Your task to perform on an android device: Add "razer blade" to the cart on bestbuy, then select checkout. Image 0: 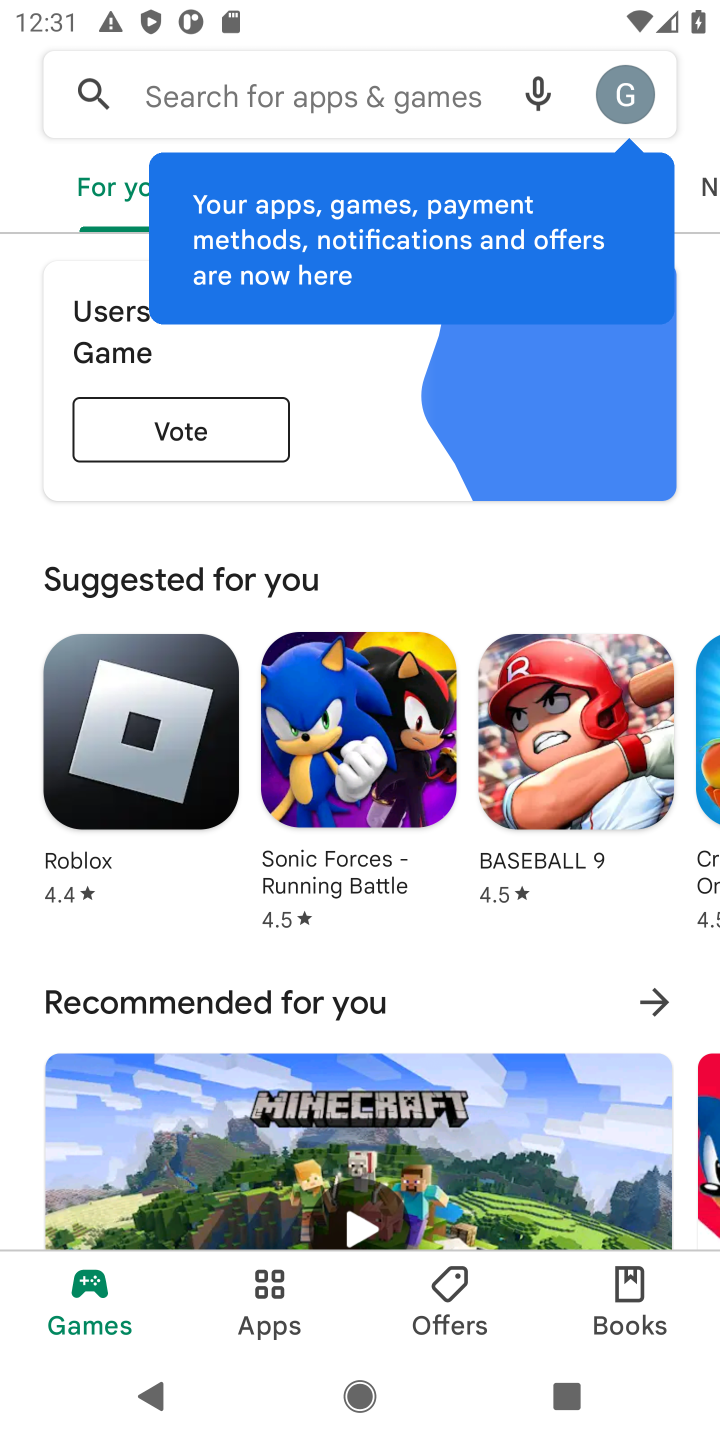
Step 0: press home button
Your task to perform on an android device: Add "razer blade" to the cart on bestbuy, then select checkout. Image 1: 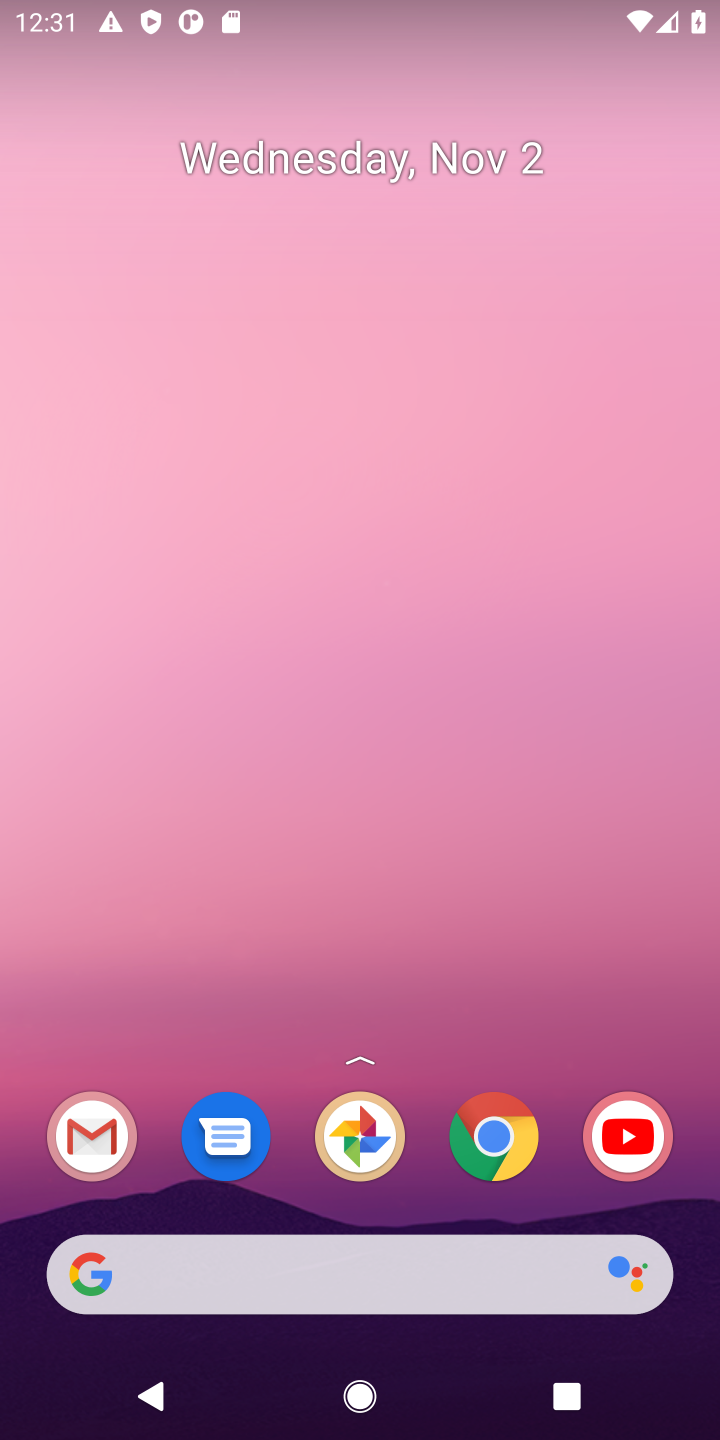
Step 1: click (493, 1150)
Your task to perform on an android device: Add "razer blade" to the cart on bestbuy, then select checkout. Image 2: 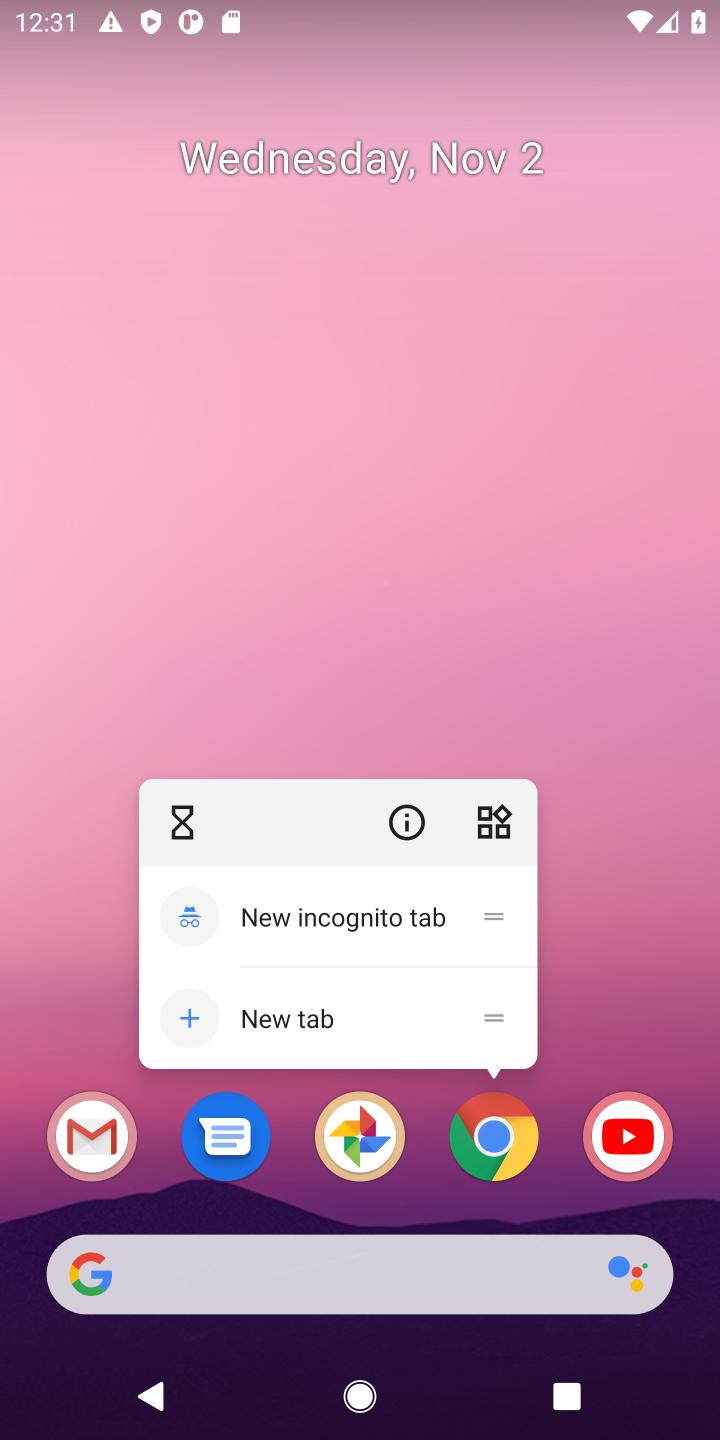
Step 2: click (490, 1142)
Your task to perform on an android device: Add "razer blade" to the cart on bestbuy, then select checkout. Image 3: 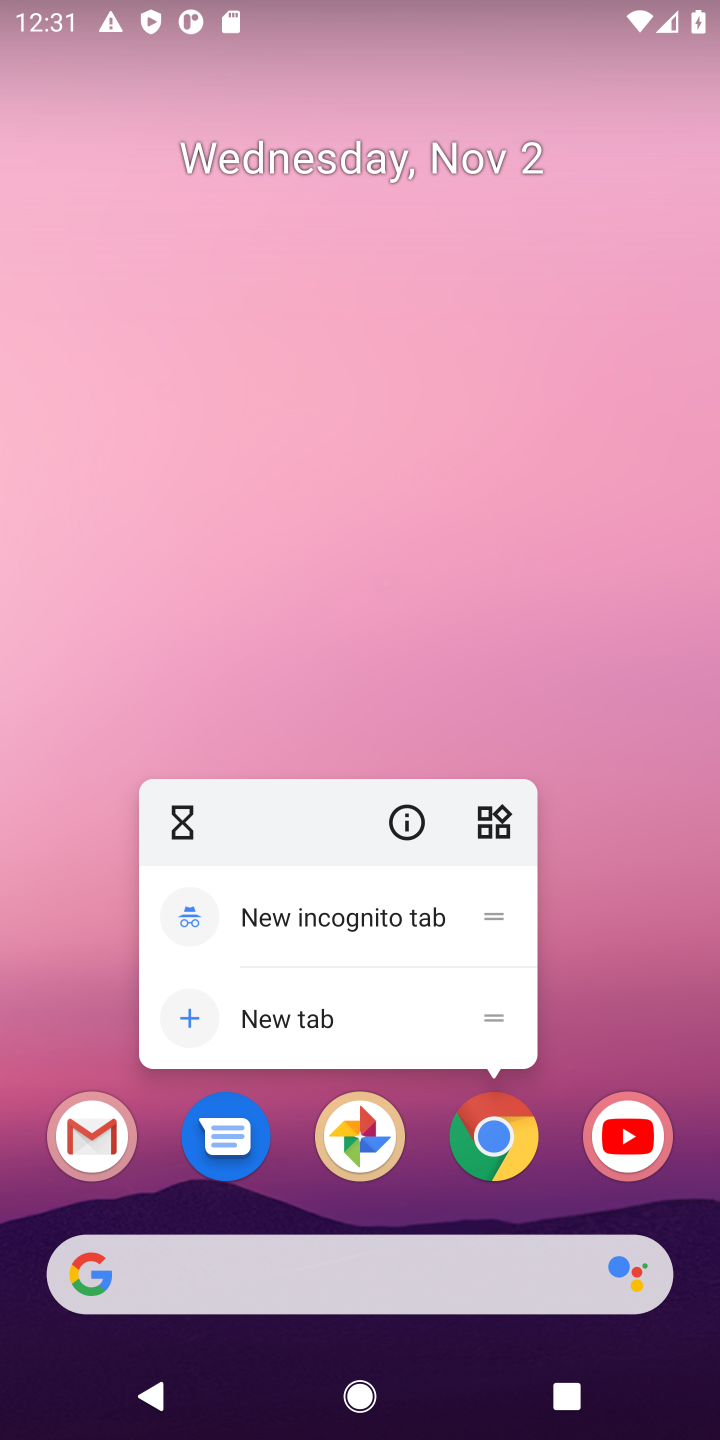
Step 3: click (494, 1136)
Your task to perform on an android device: Add "razer blade" to the cart on bestbuy, then select checkout. Image 4: 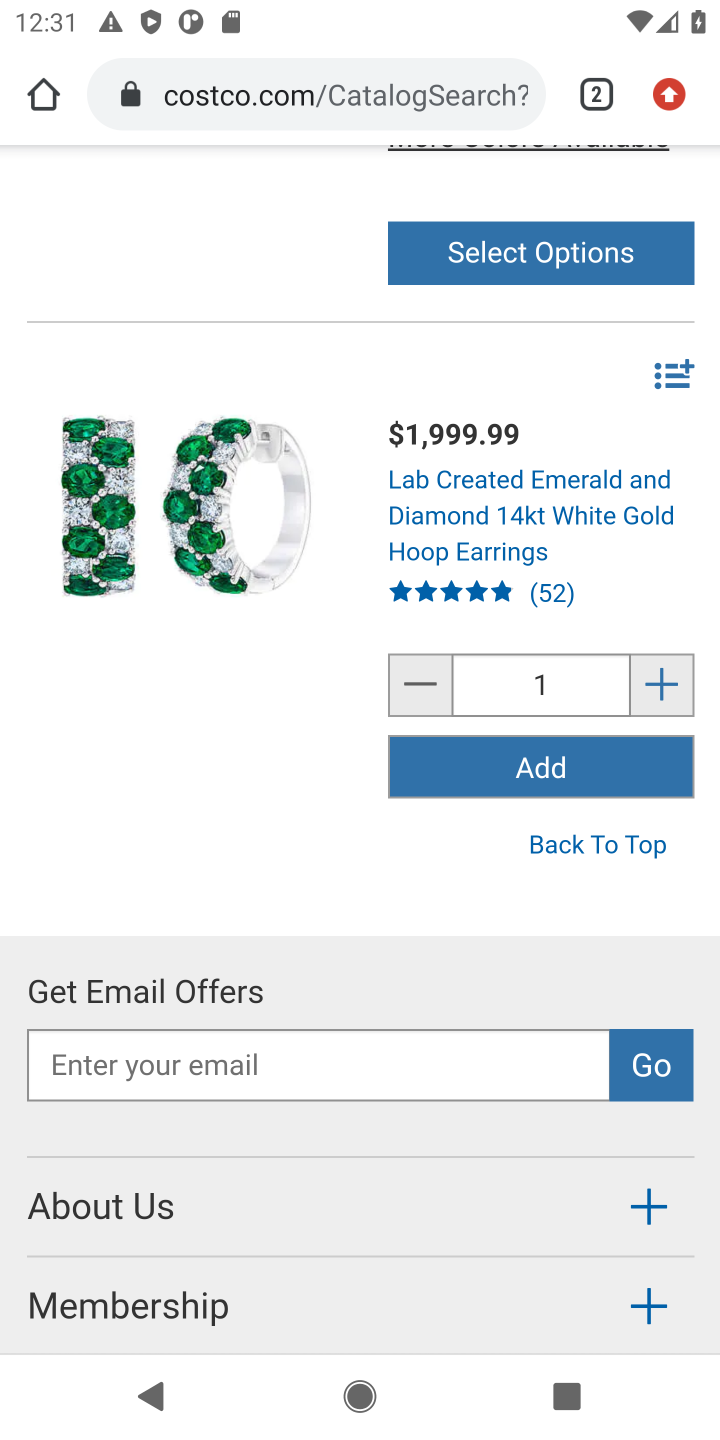
Step 4: click (342, 88)
Your task to perform on an android device: Add "razer blade" to the cart on bestbuy, then select checkout. Image 5: 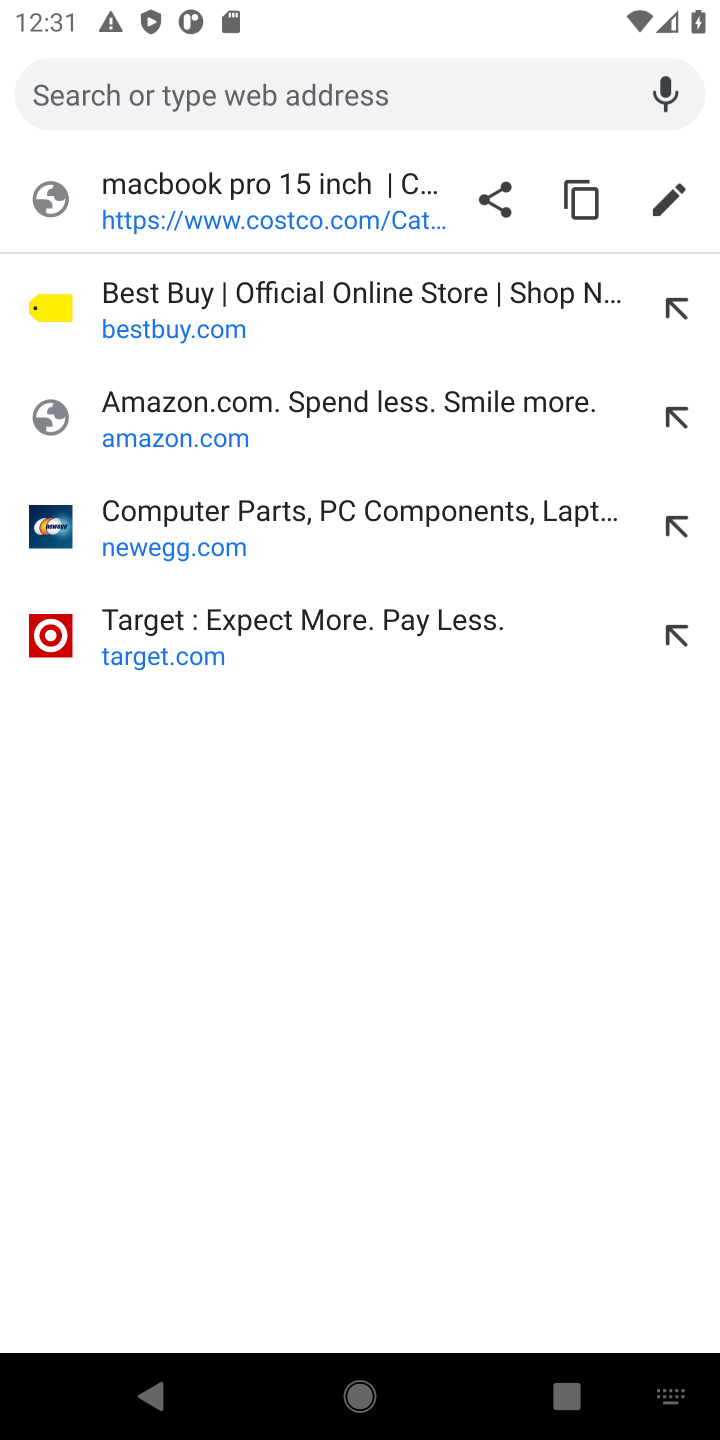
Step 5: type "bestbuy"
Your task to perform on an android device: Add "razer blade" to the cart on bestbuy, then select checkout. Image 6: 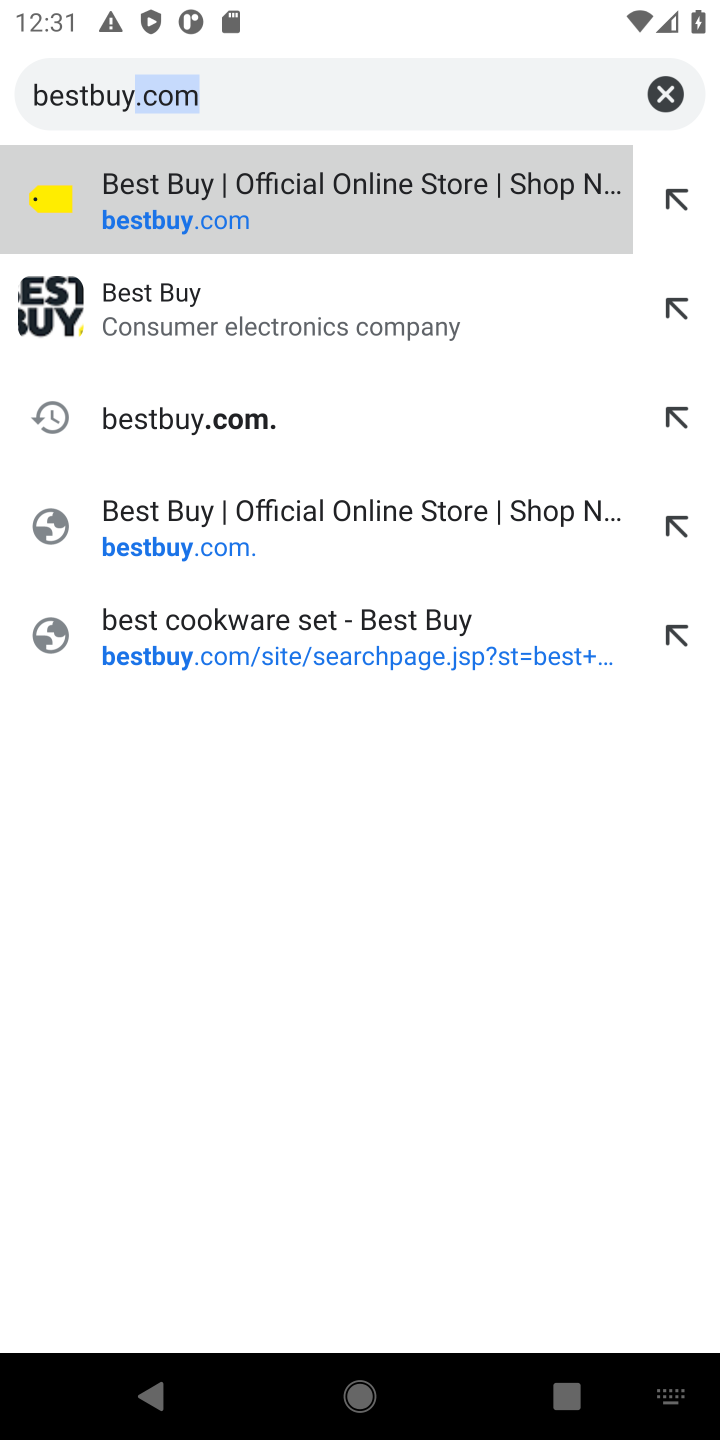
Step 6: click (537, 208)
Your task to perform on an android device: Add "razer blade" to the cart on bestbuy, then select checkout. Image 7: 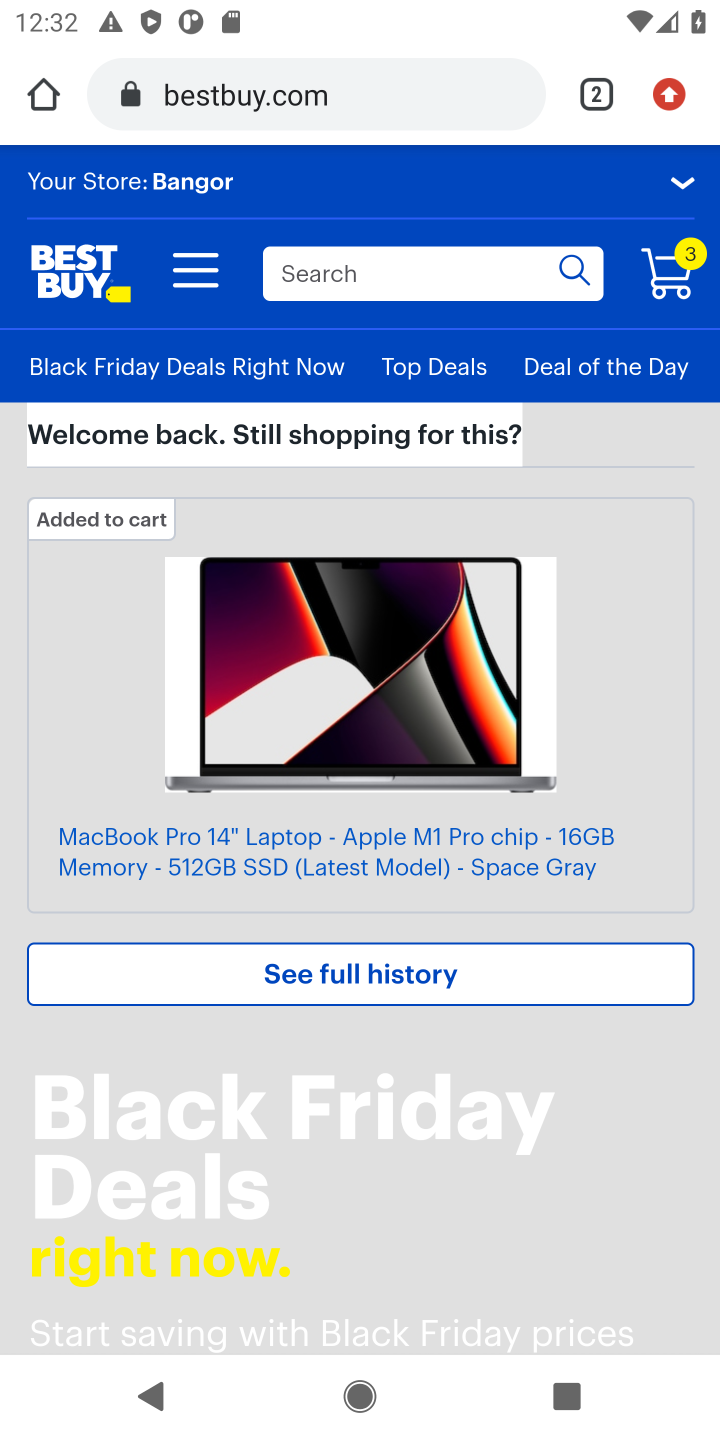
Step 7: click (362, 225)
Your task to perform on an android device: Add "razer blade" to the cart on bestbuy, then select checkout. Image 8: 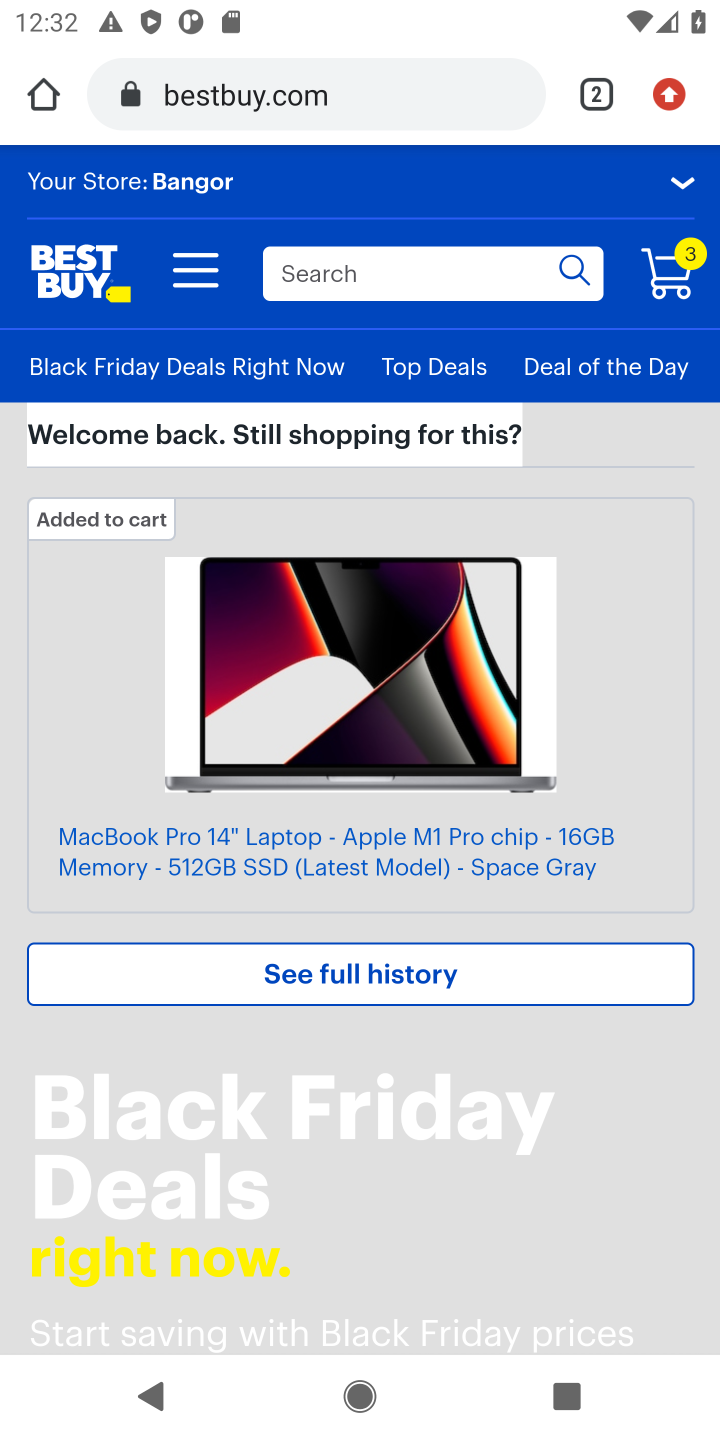
Step 8: click (350, 252)
Your task to perform on an android device: Add "razer blade" to the cart on bestbuy, then select checkout. Image 9: 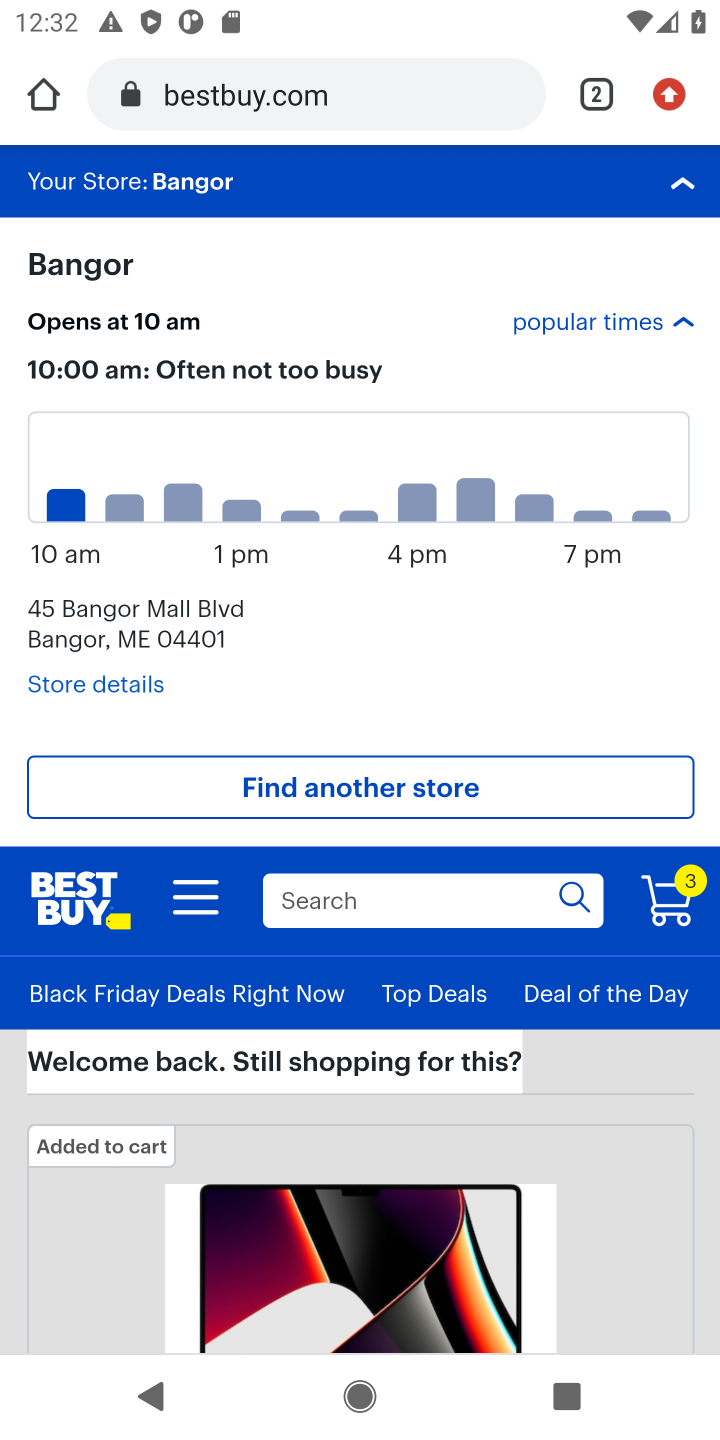
Step 9: click (319, 913)
Your task to perform on an android device: Add "razer blade" to the cart on bestbuy, then select checkout. Image 10: 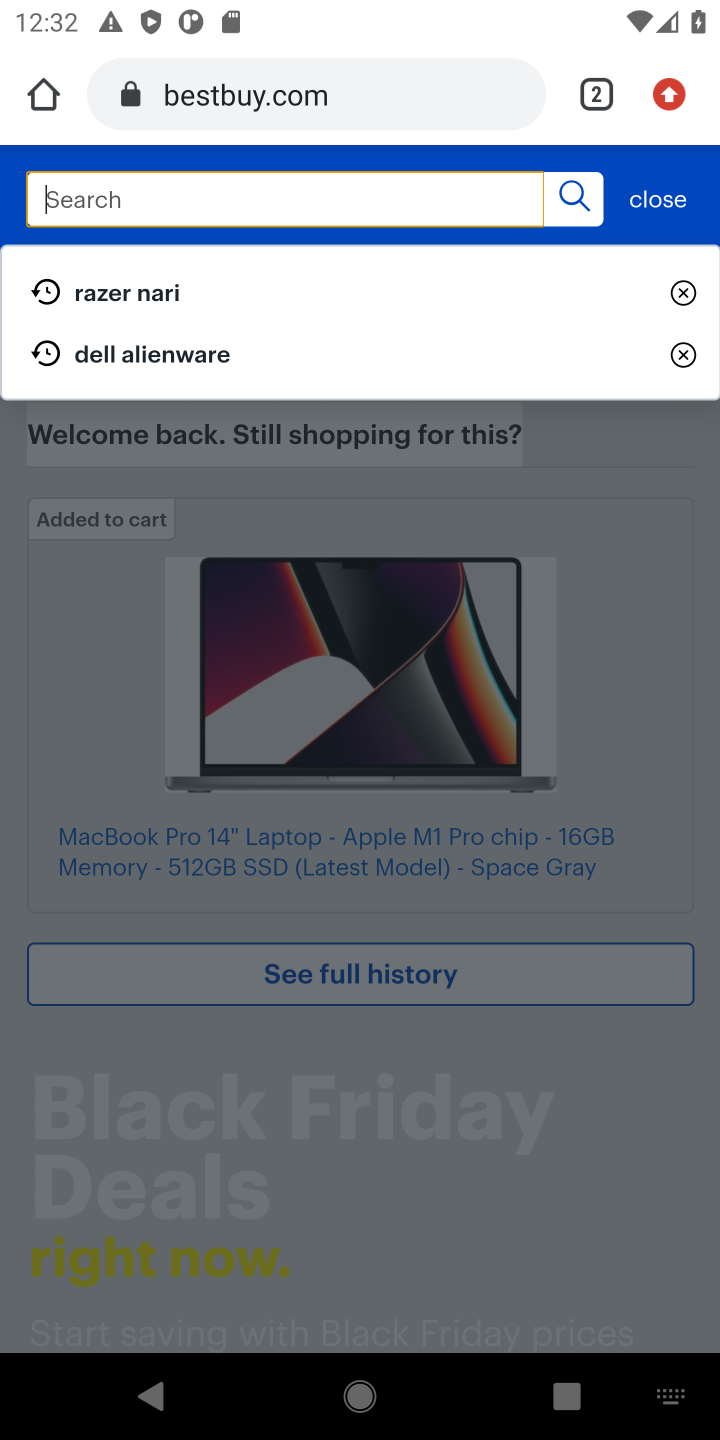
Step 10: type "razer blade"
Your task to perform on an android device: Add "razer blade" to the cart on bestbuy, then select checkout. Image 11: 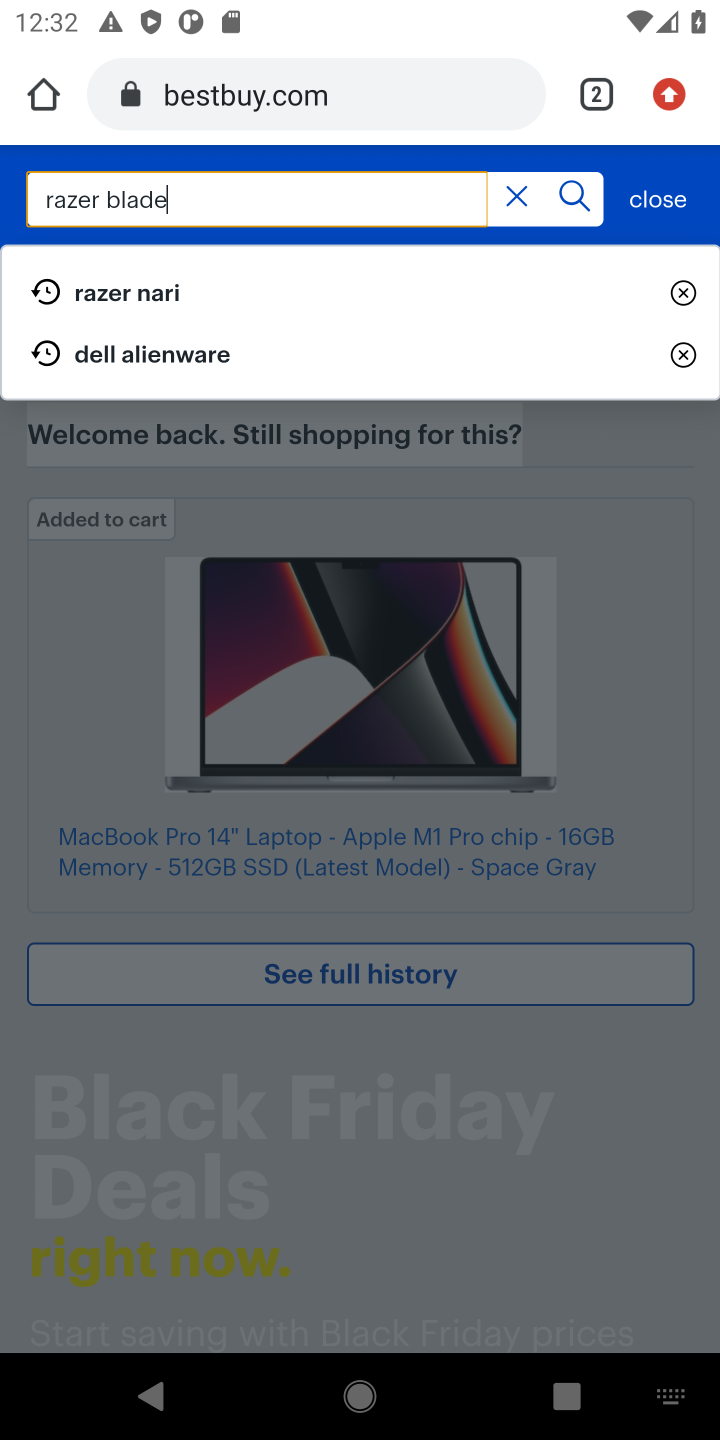
Step 11: type ""
Your task to perform on an android device: Add "razer blade" to the cart on bestbuy, then select checkout. Image 12: 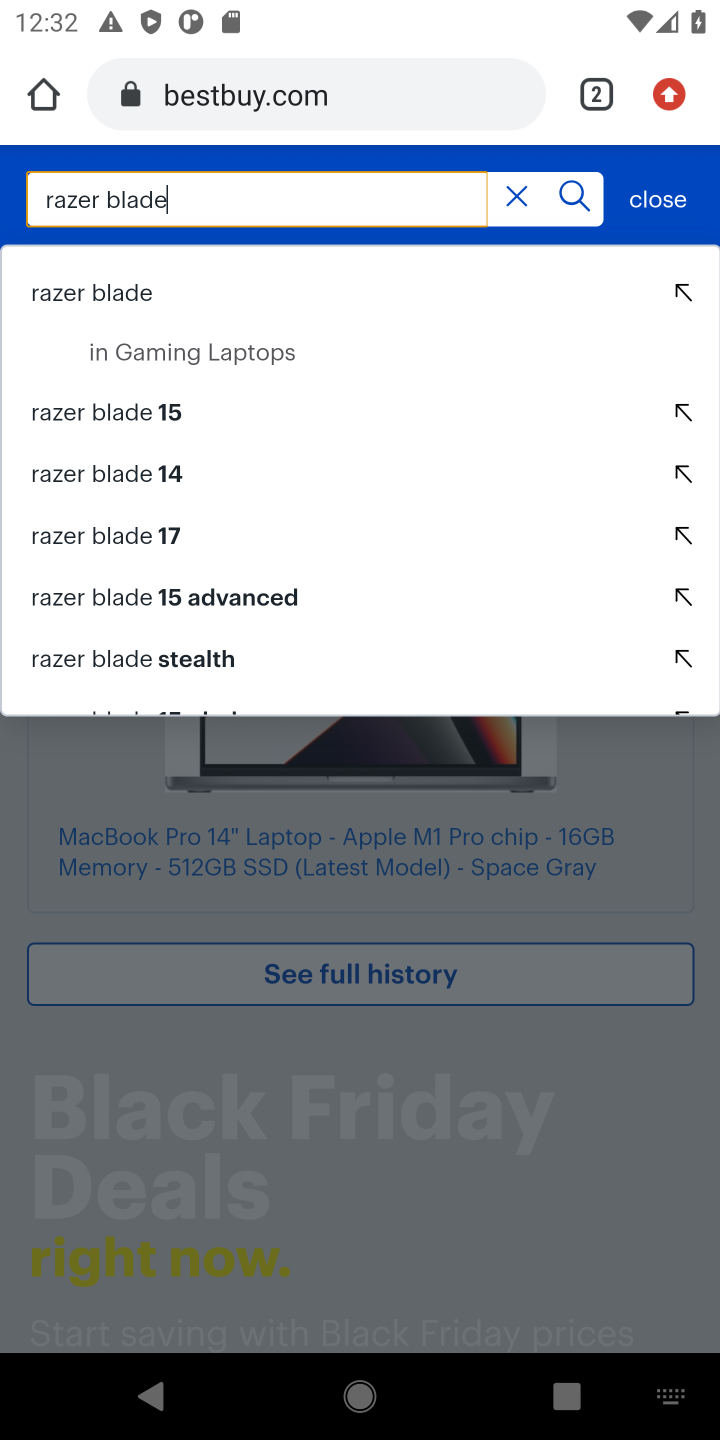
Step 12: click (571, 190)
Your task to perform on an android device: Add "razer blade" to the cart on bestbuy, then select checkout. Image 13: 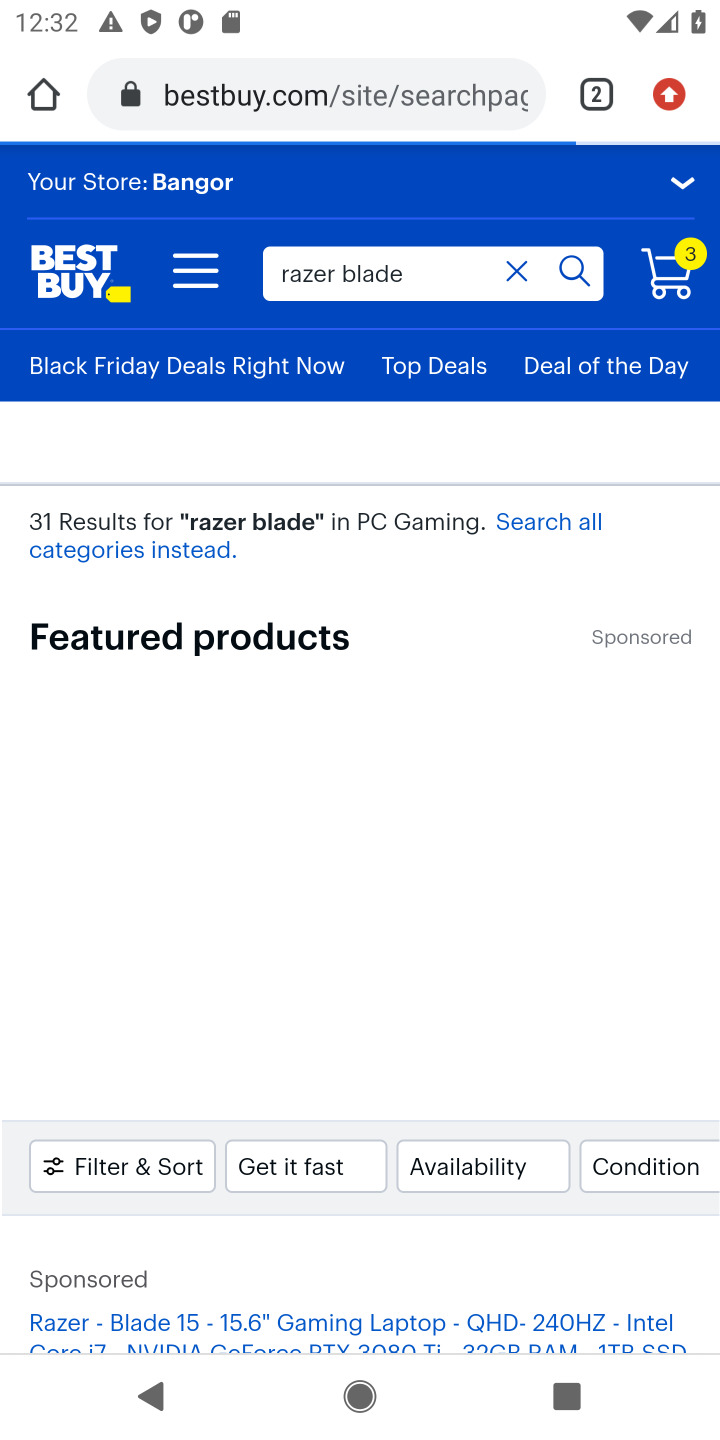
Step 13: drag from (490, 826) to (626, 445)
Your task to perform on an android device: Add "razer blade" to the cart on bestbuy, then select checkout. Image 14: 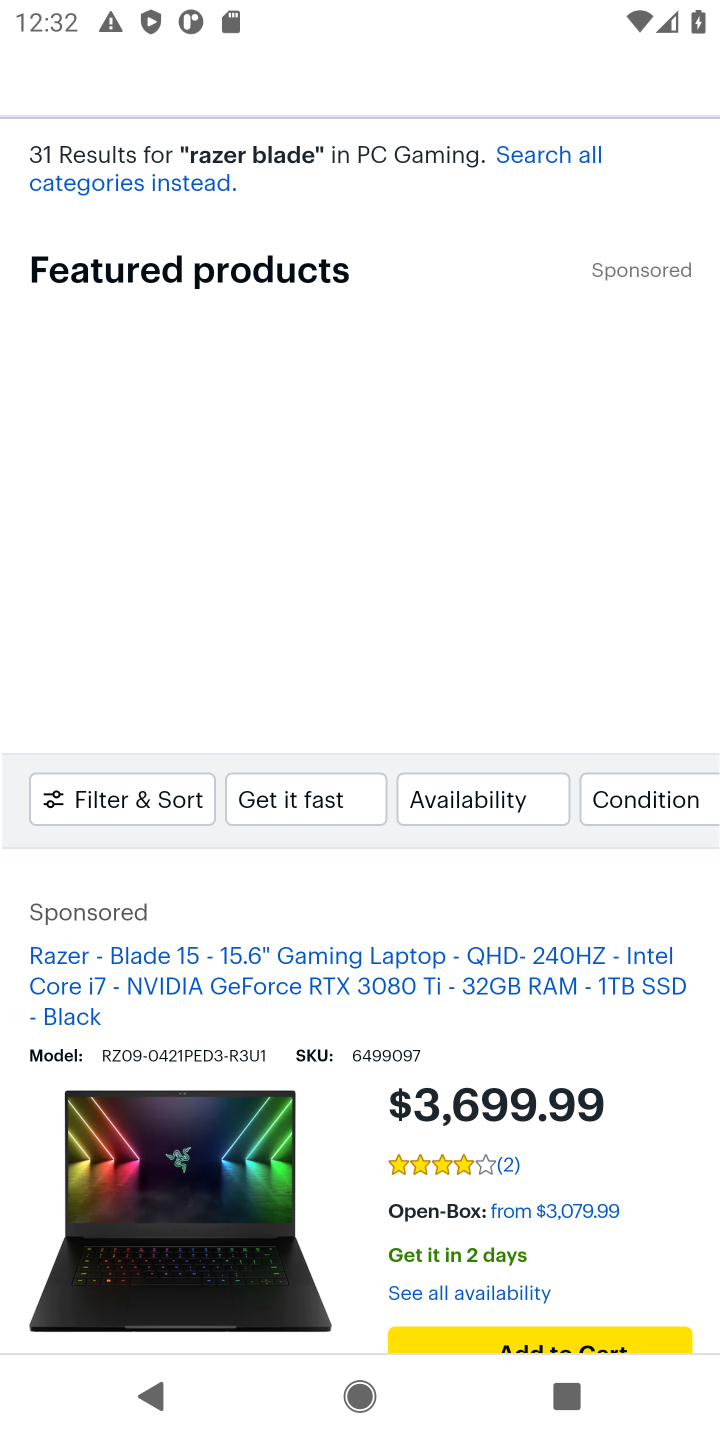
Step 14: drag from (369, 1018) to (429, 746)
Your task to perform on an android device: Add "razer blade" to the cart on bestbuy, then select checkout. Image 15: 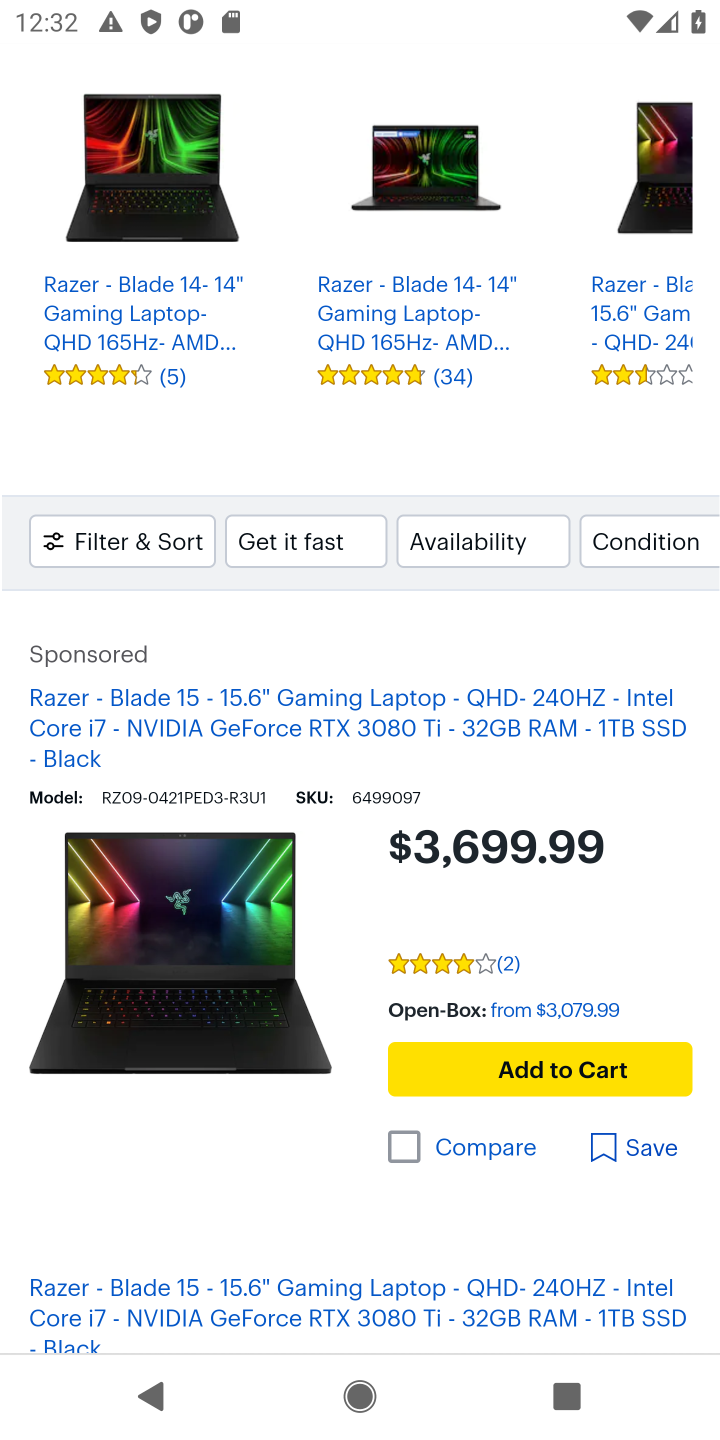
Step 15: click (520, 1021)
Your task to perform on an android device: Add "razer blade" to the cart on bestbuy, then select checkout. Image 16: 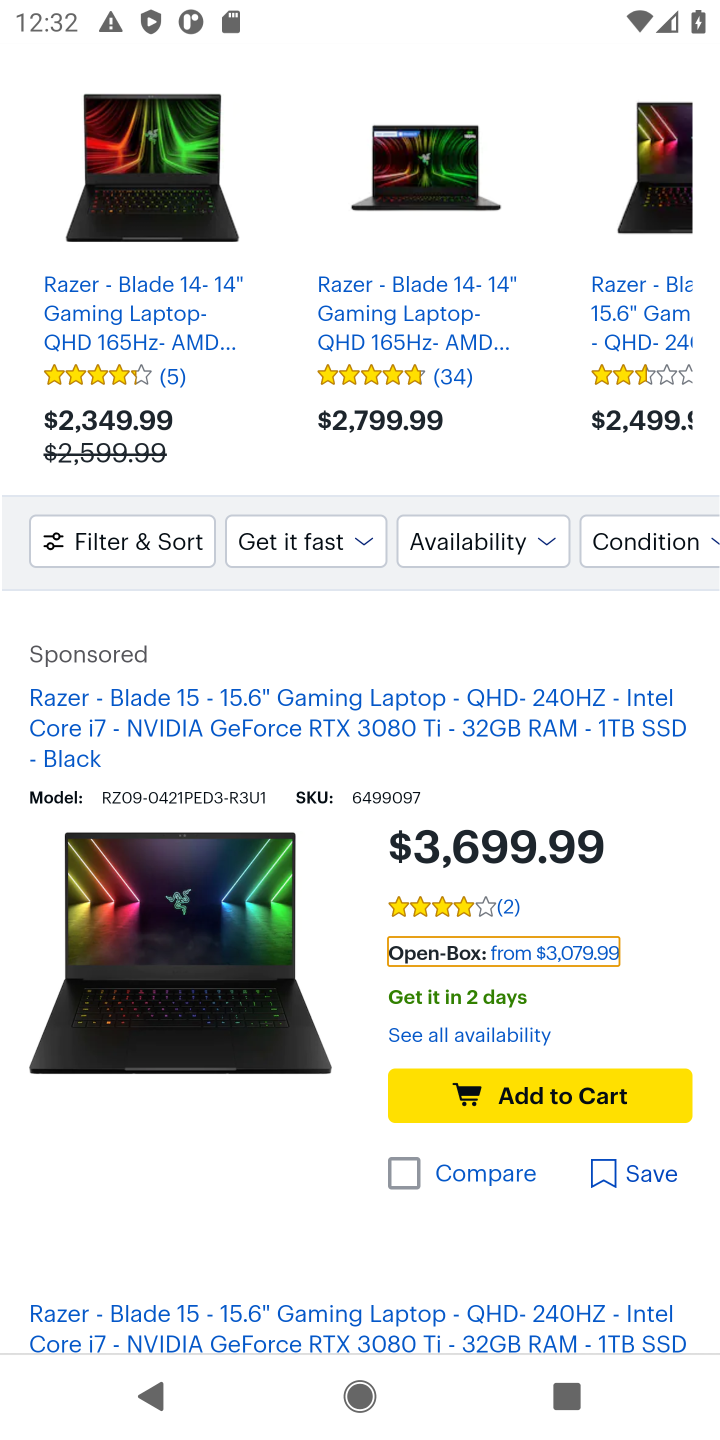
Step 16: click (499, 1167)
Your task to perform on an android device: Add "razer blade" to the cart on bestbuy, then select checkout. Image 17: 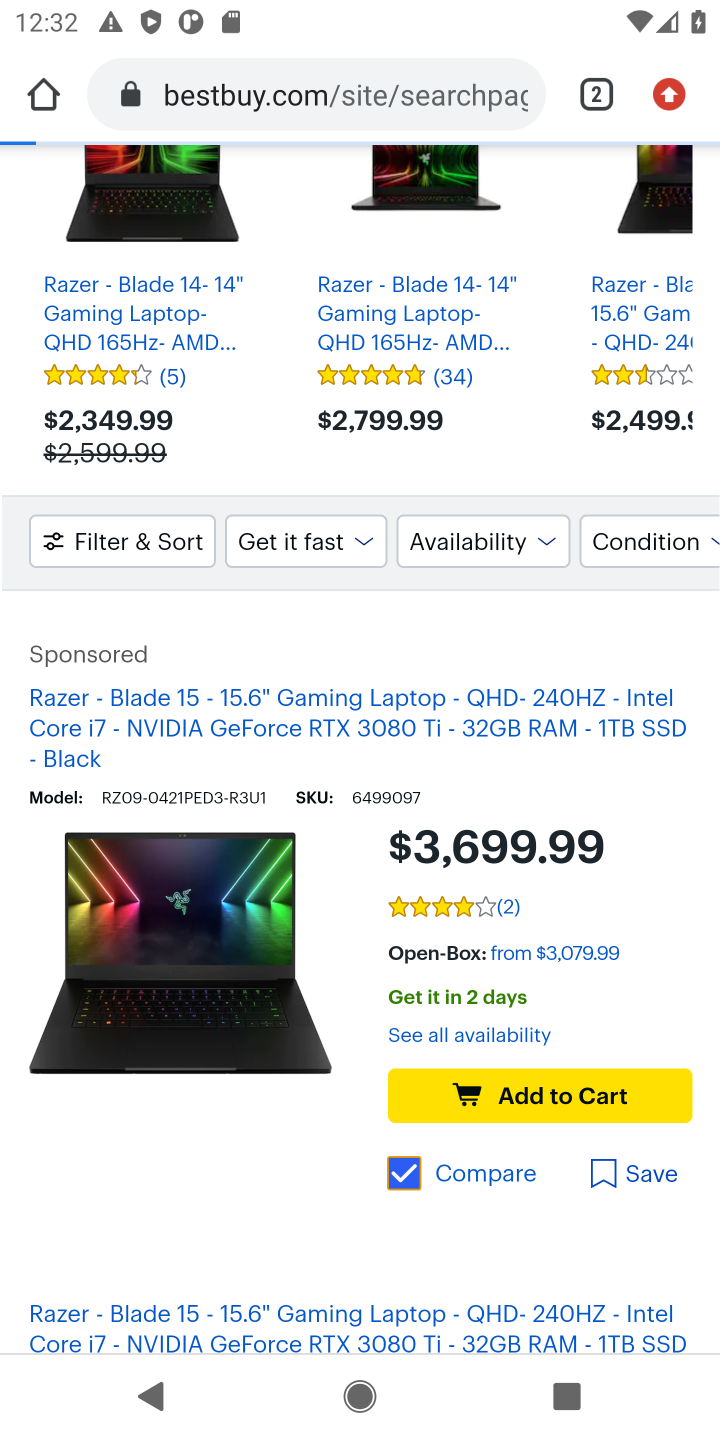
Step 17: click (521, 1092)
Your task to perform on an android device: Add "razer blade" to the cart on bestbuy, then select checkout. Image 18: 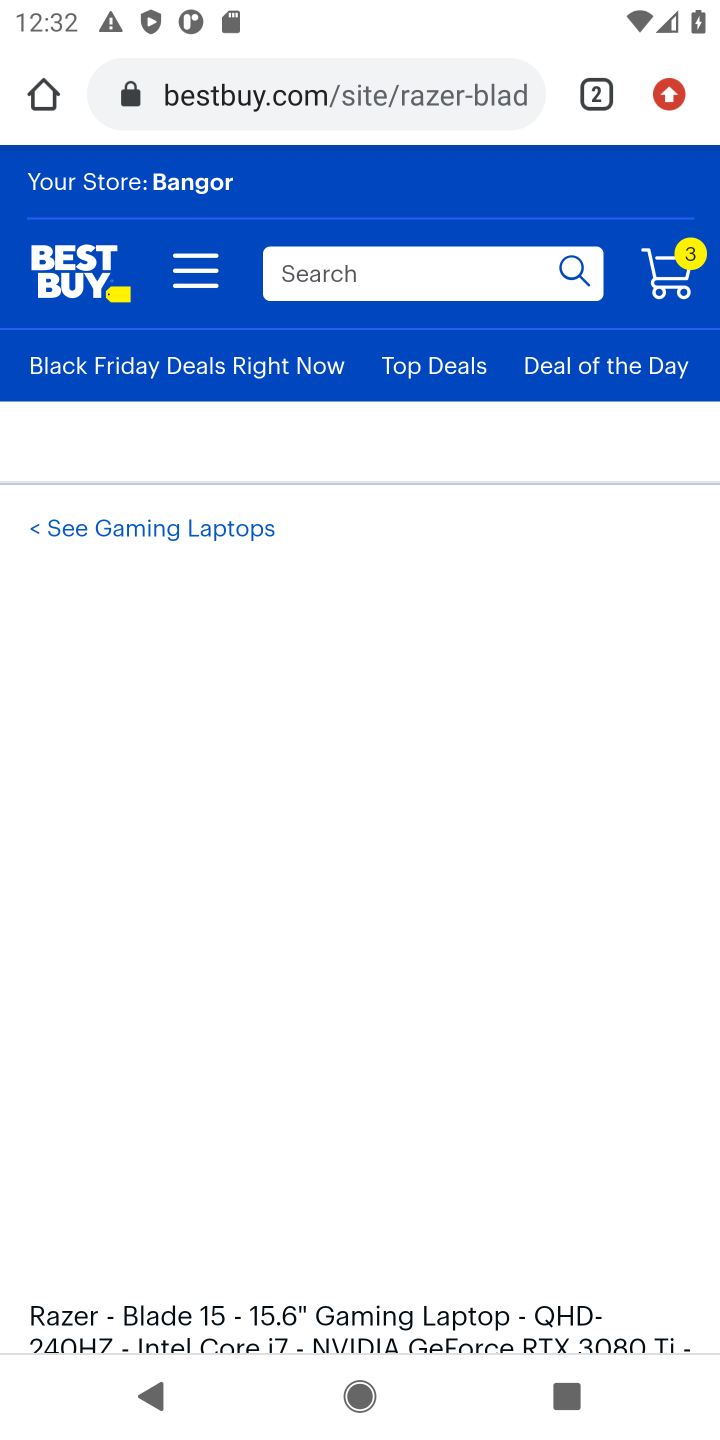
Step 18: click (693, 274)
Your task to perform on an android device: Add "razer blade" to the cart on bestbuy, then select checkout. Image 19: 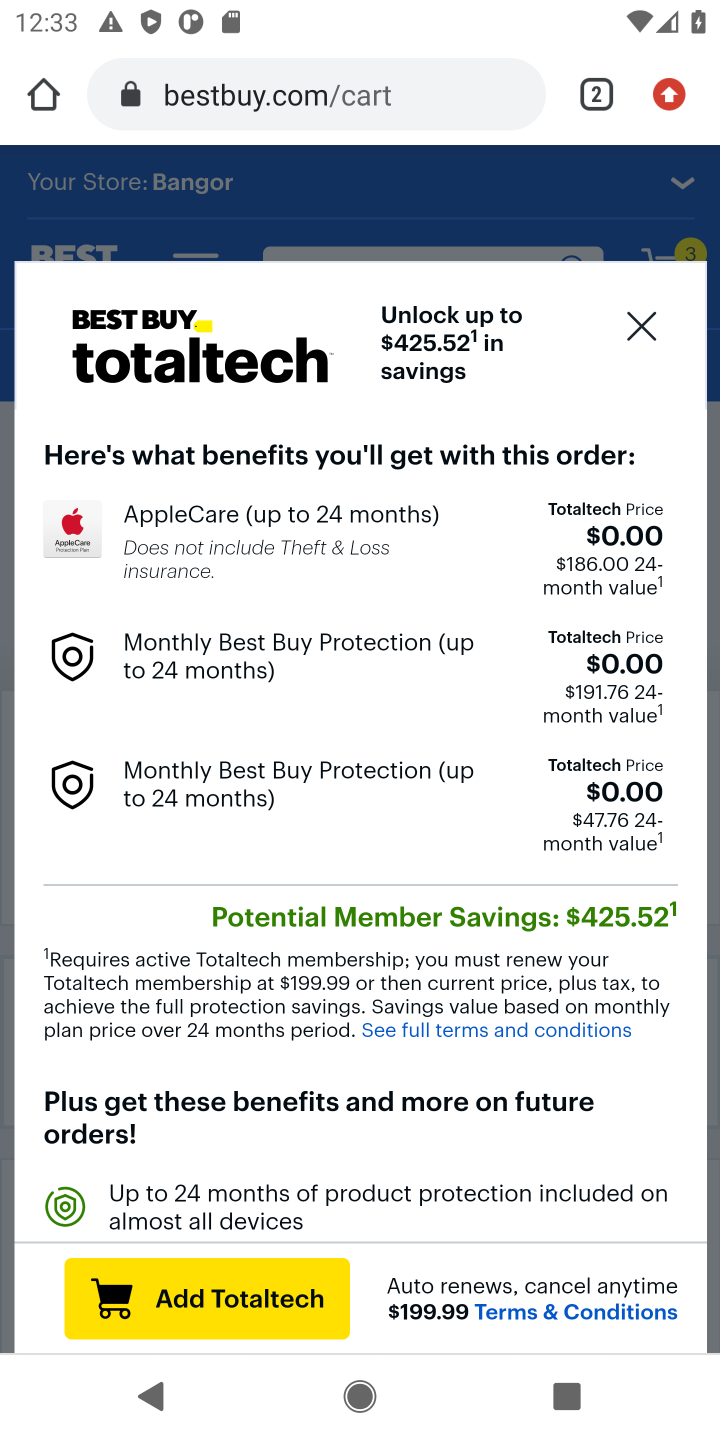
Step 19: click (651, 321)
Your task to perform on an android device: Add "razer blade" to the cart on bestbuy, then select checkout. Image 20: 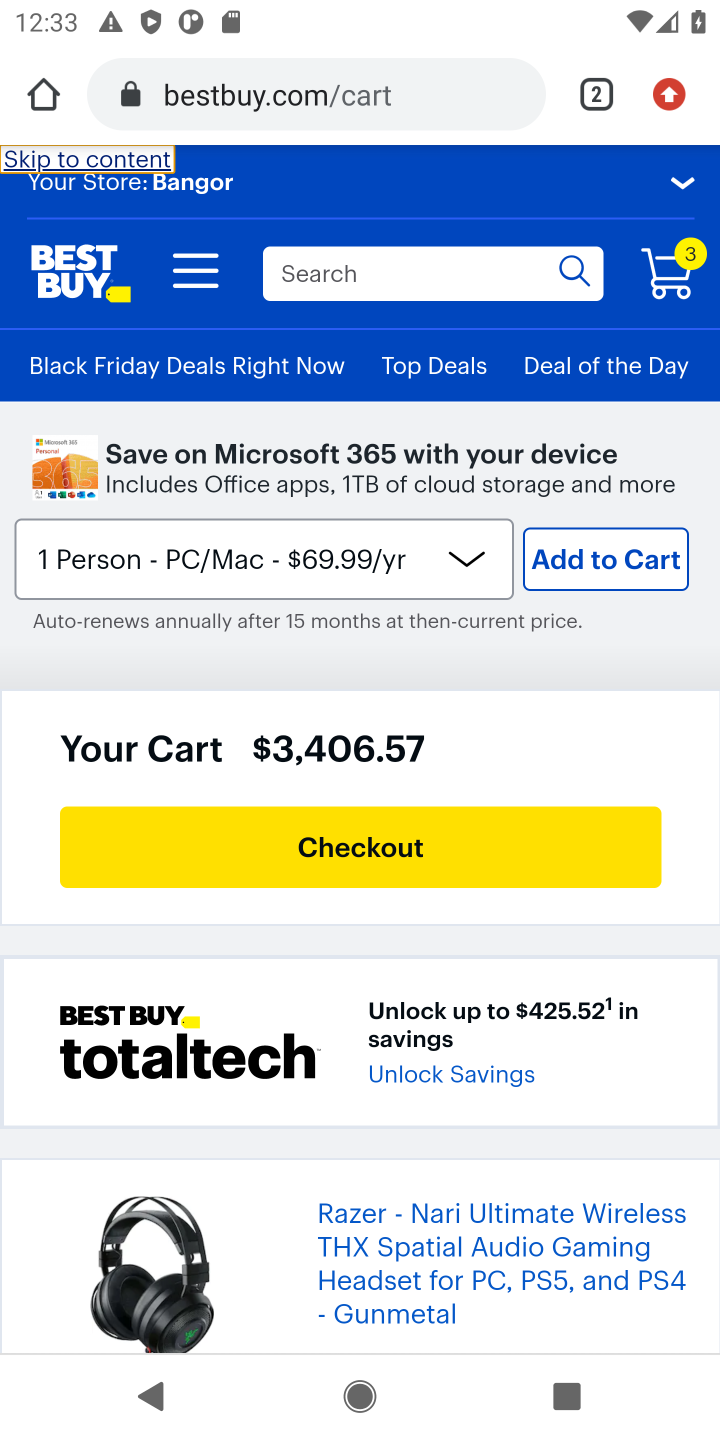
Step 20: drag from (446, 1064) to (520, 410)
Your task to perform on an android device: Add "razer blade" to the cart on bestbuy, then select checkout. Image 21: 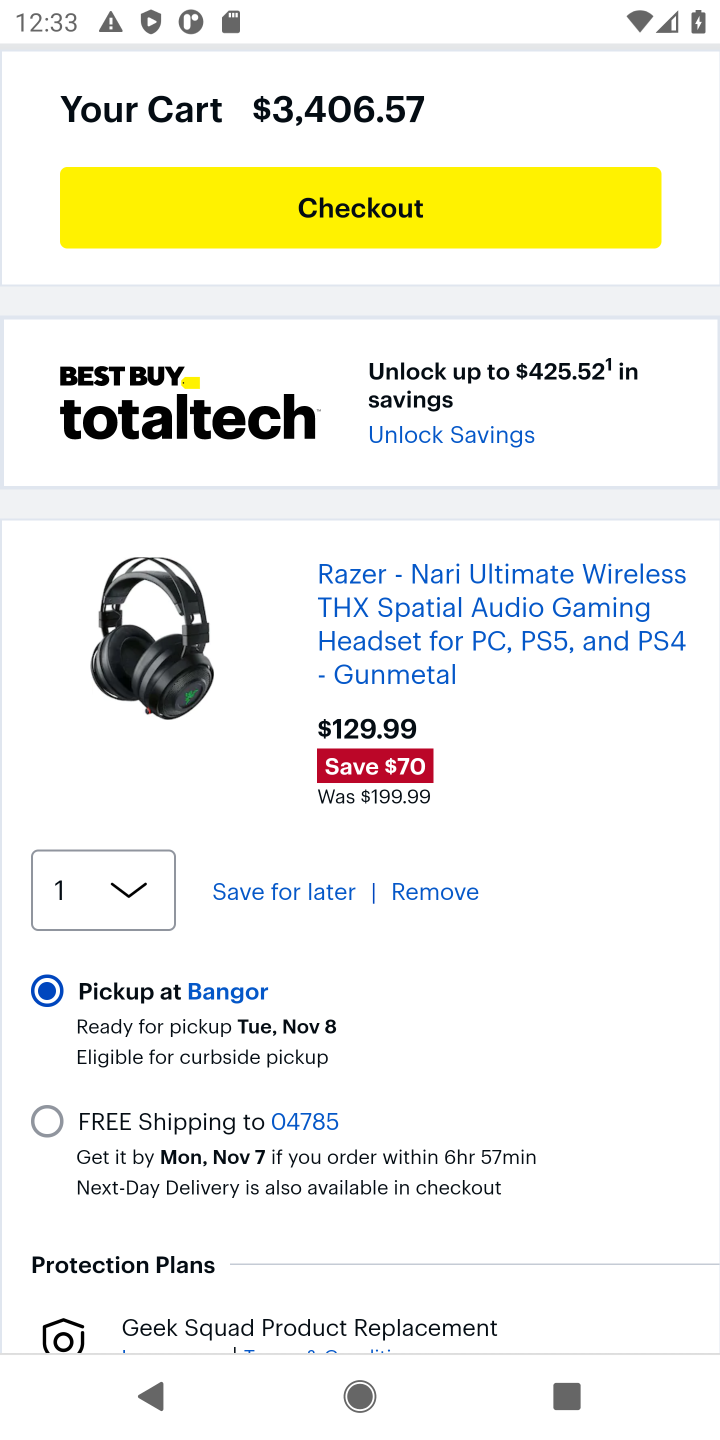
Step 21: click (139, 860)
Your task to perform on an android device: Add "razer blade" to the cart on bestbuy, then select checkout. Image 22: 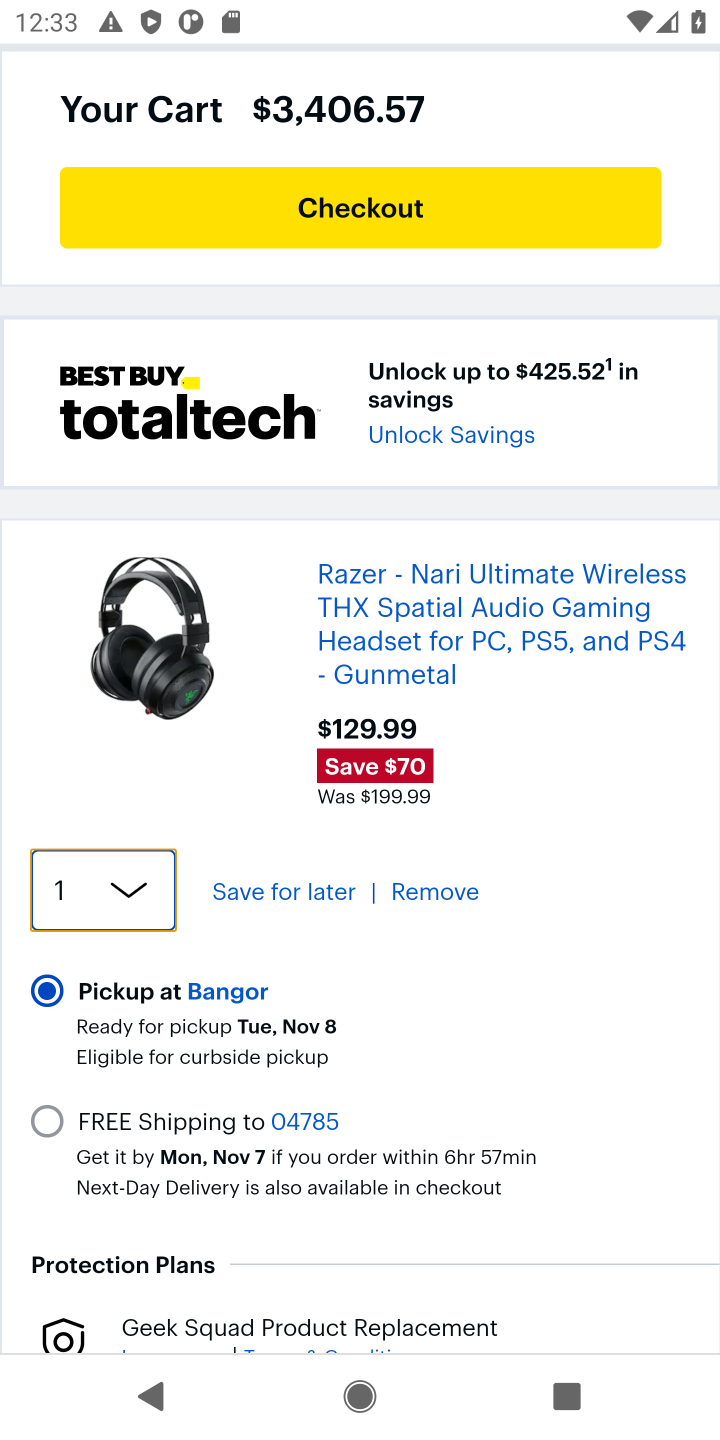
Step 22: click (128, 885)
Your task to perform on an android device: Add "razer blade" to the cart on bestbuy, then select checkout. Image 23: 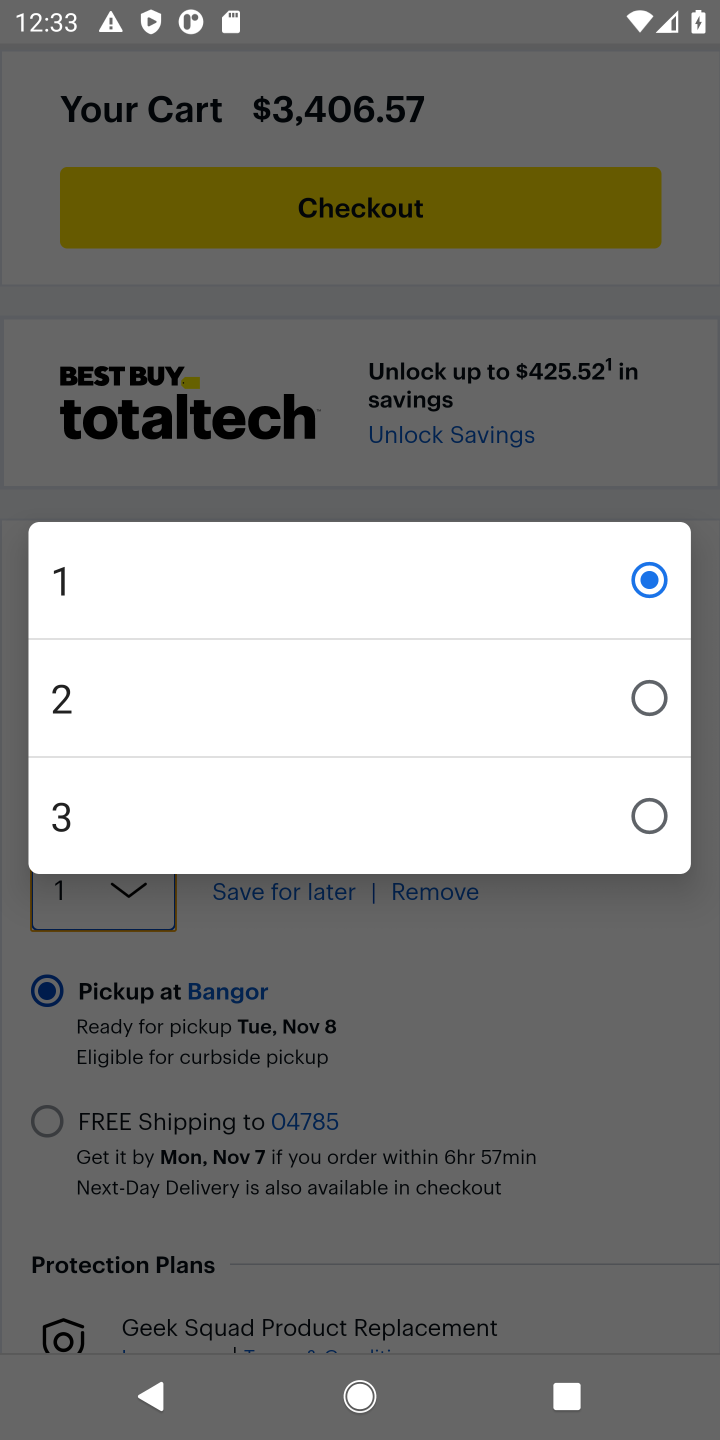
Step 23: click (248, 467)
Your task to perform on an android device: Add "razer blade" to the cart on bestbuy, then select checkout. Image 24: 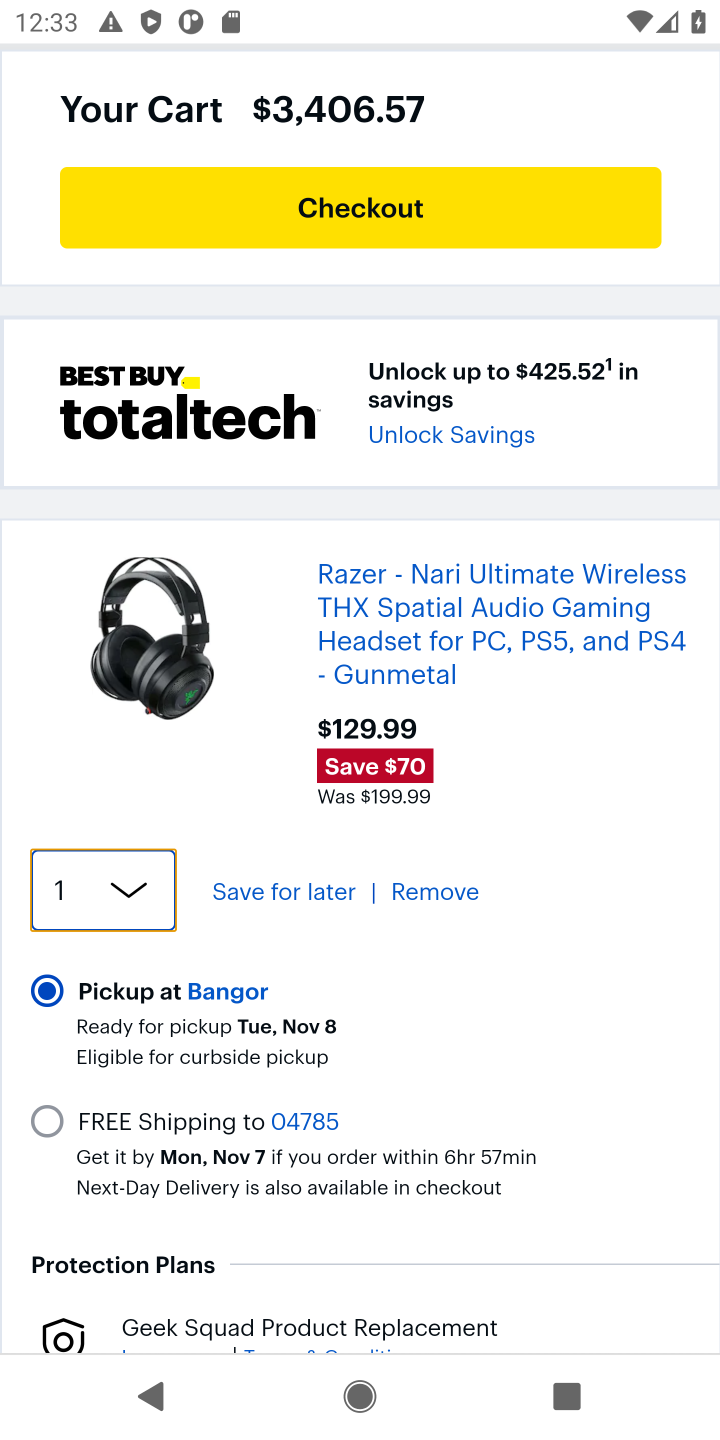
Step 24: click (407, 142)
Your task to perform on an android device: Add "razer blade" to the cart on bestbuy, then select checkout. Image 25: 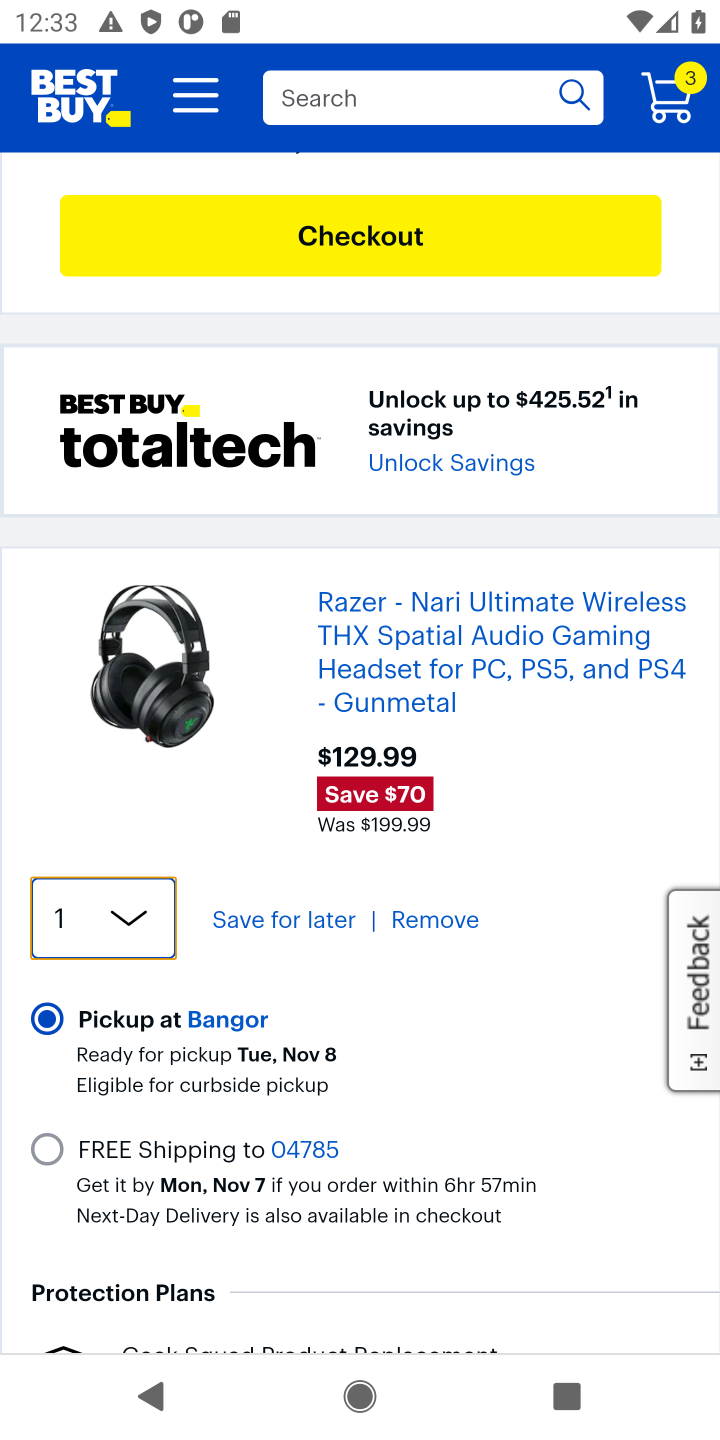
Step 25: click (376, 234)
Your task to perform on an android device: Add "razer blade" to the cart on bestbuy, then select checkout. Image 26: 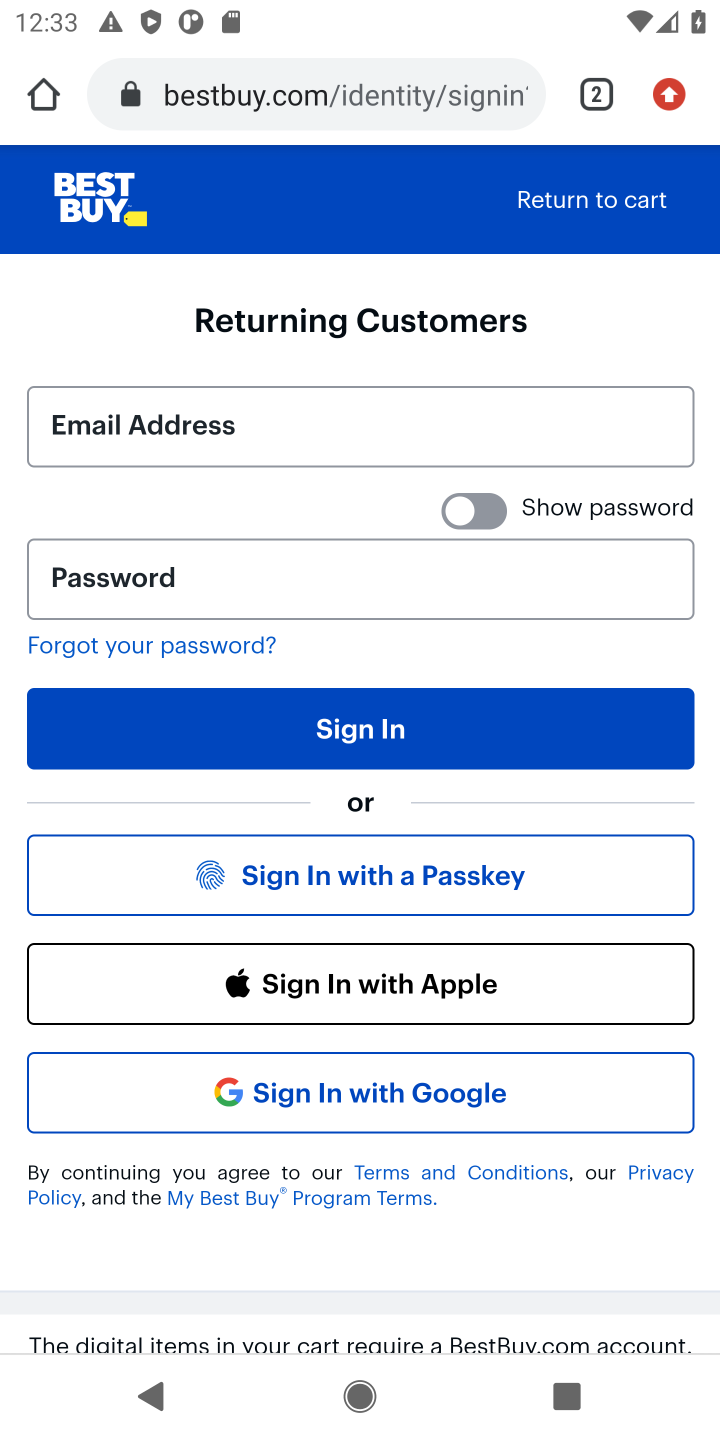
Step 26: press home button
Your task to perform on an android device: Add "razer blade" to the cart on bestbuy, then select checkout. Image 27: 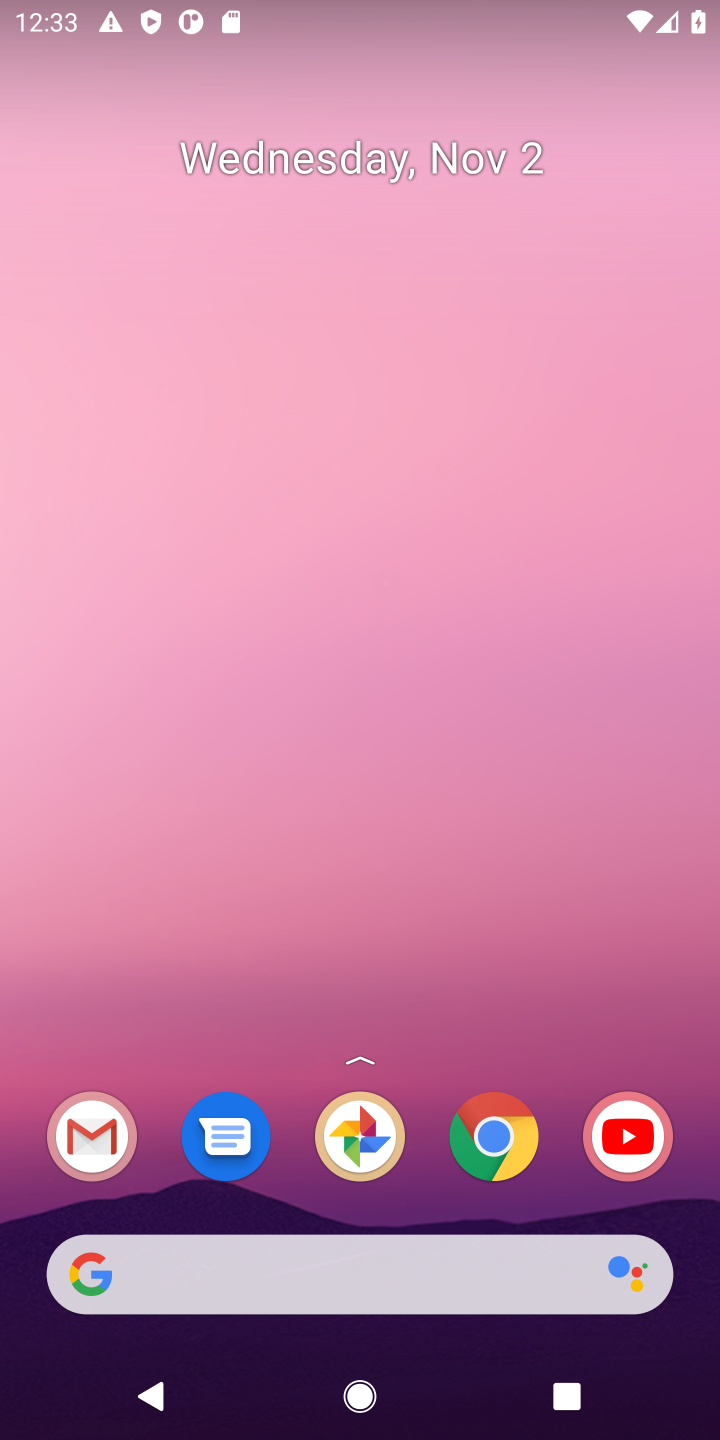
Step 27: click (503, 1149)
Your task to perform on an android device: Add "razer blade" to the cart on bestbuy, then select checkout. Image 28: 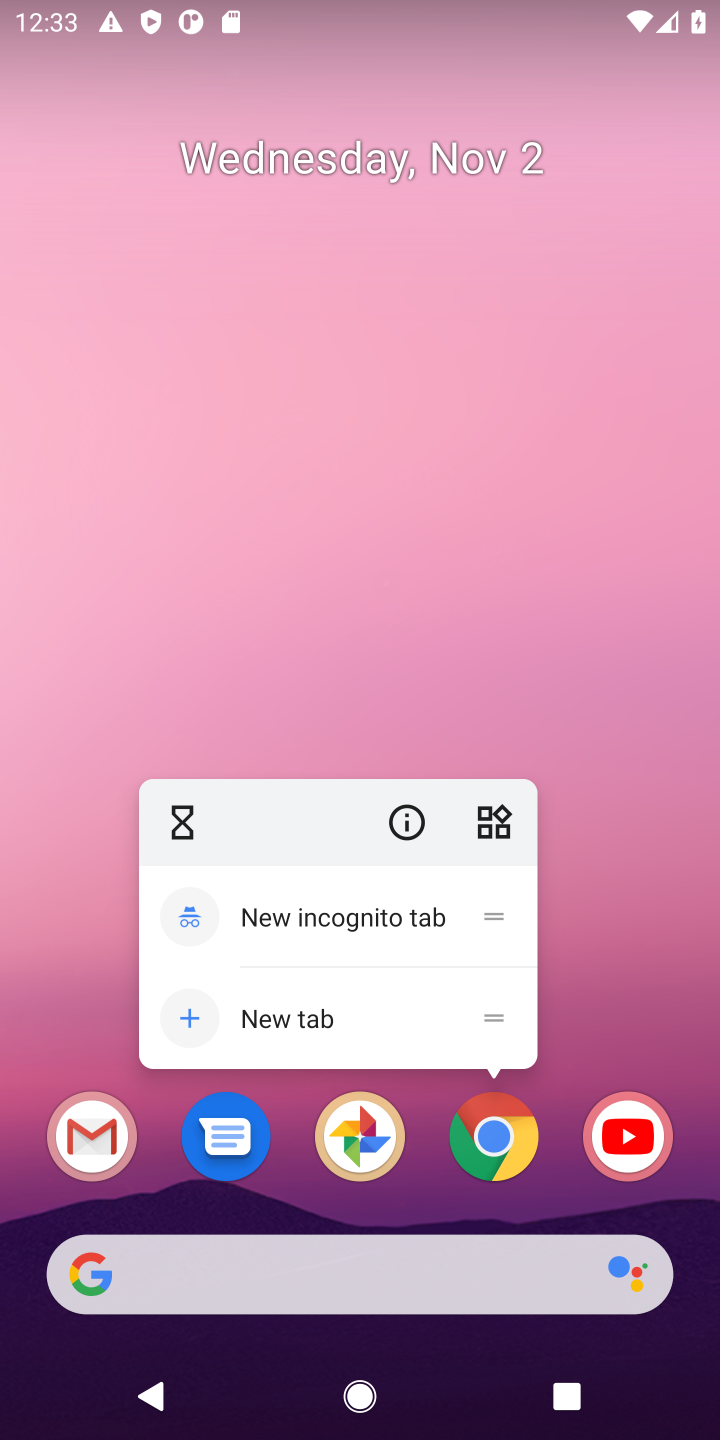
Step 28: click (499, 1140)
Your task to perform on an android device: Add "razer blade" to the cart on bestbuy, then select checkout. Image 29: 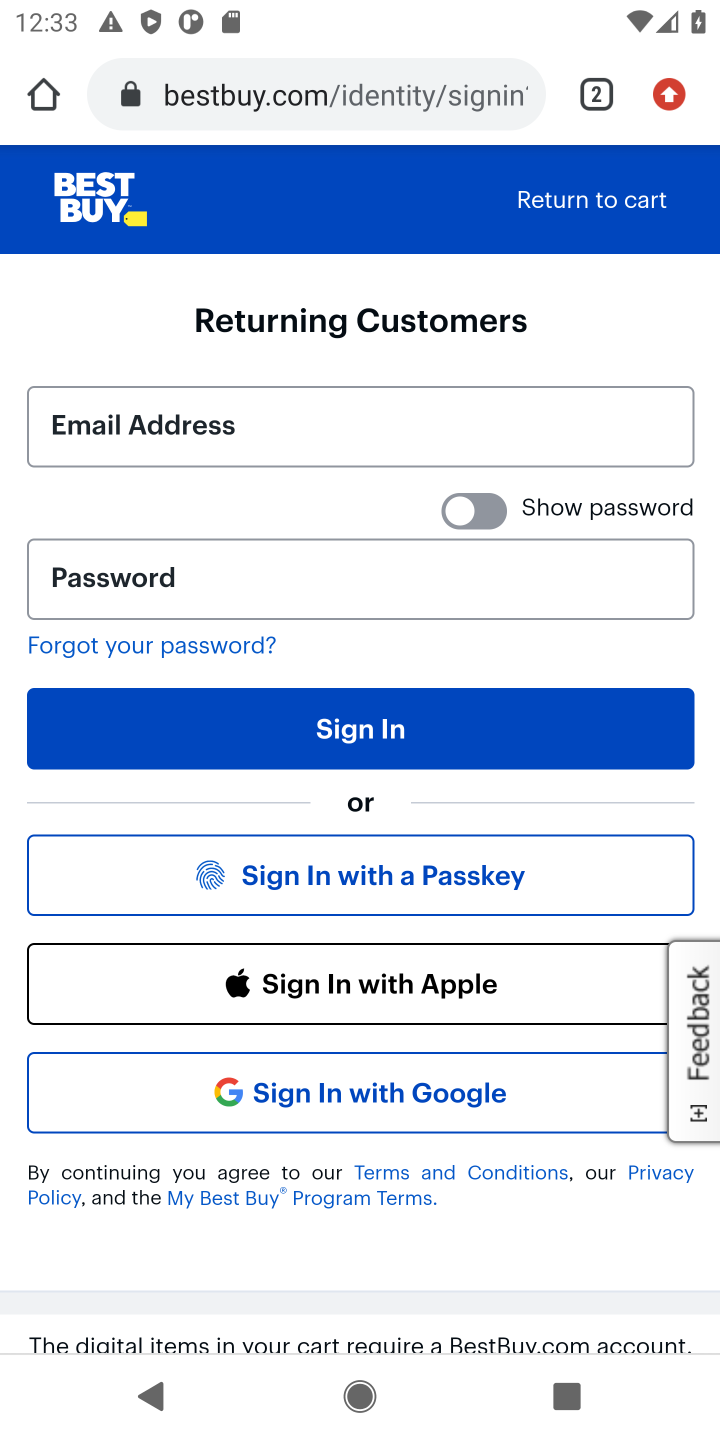
Step 29: click (219, 110)
Your task to perform on an android device: Add "razer blade" to the cart on bestbuy, then select checkout. Image 30: 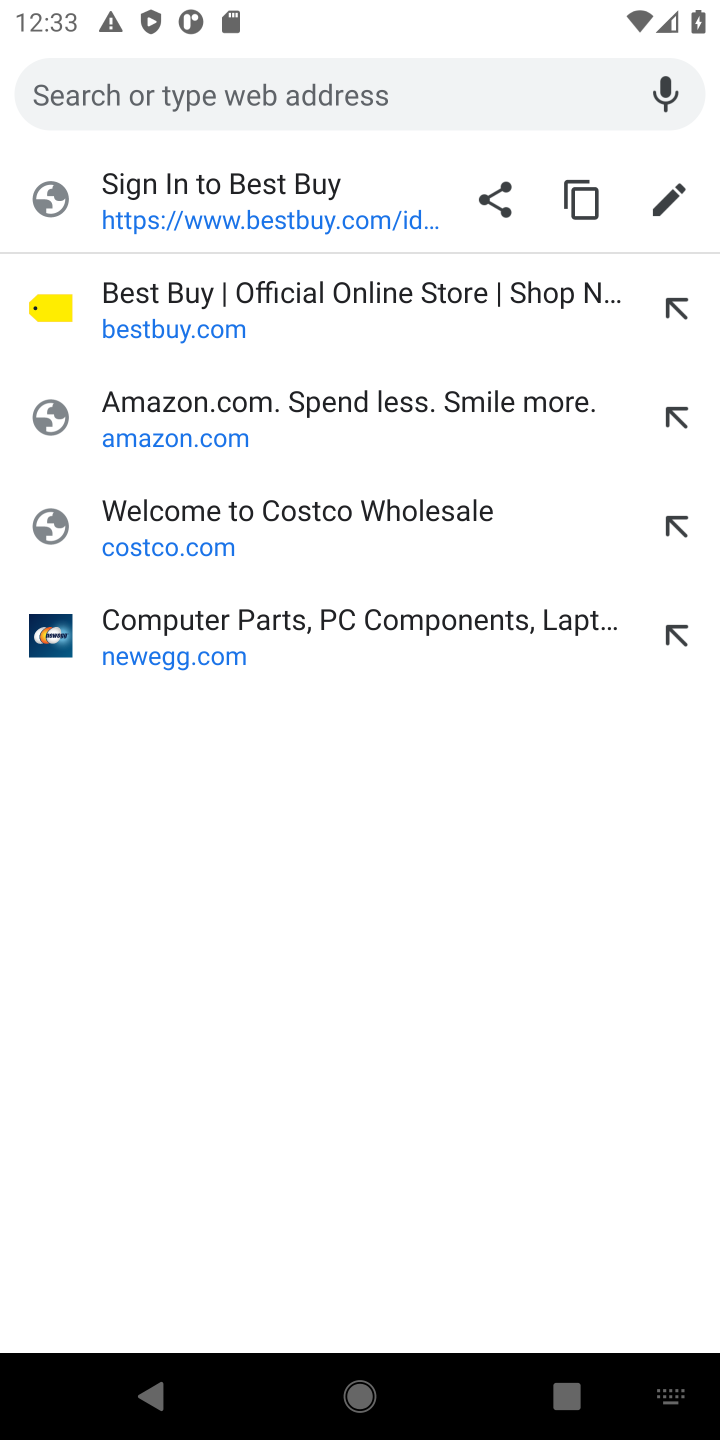
Step 30: type "bestbuy"
Your task to perform on an android device: Add "razer blade" to the cart on bestbuy, then select checkout. Image 31: 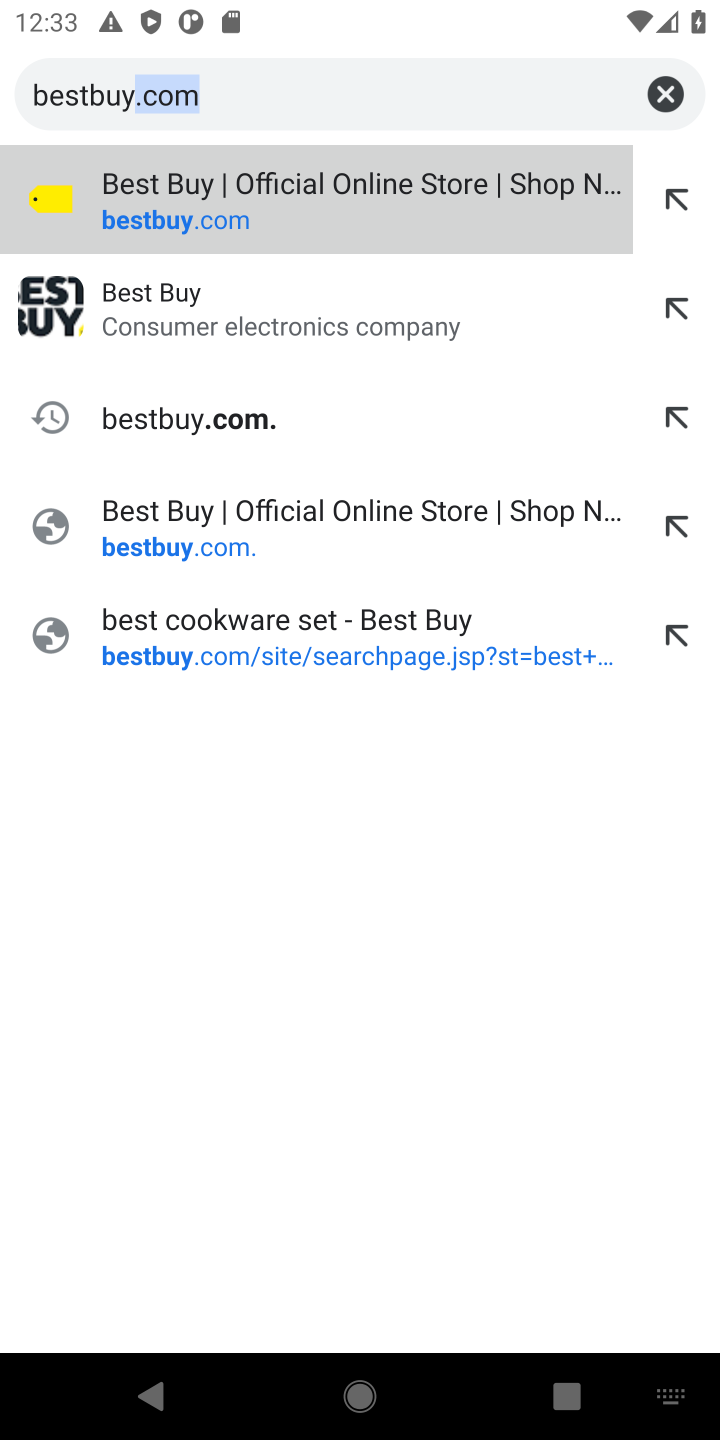
Step 31: type ""
Your task to perform on an android device: Add "razer blade" to the cart on bestbuy, then select checkout. Image 32: 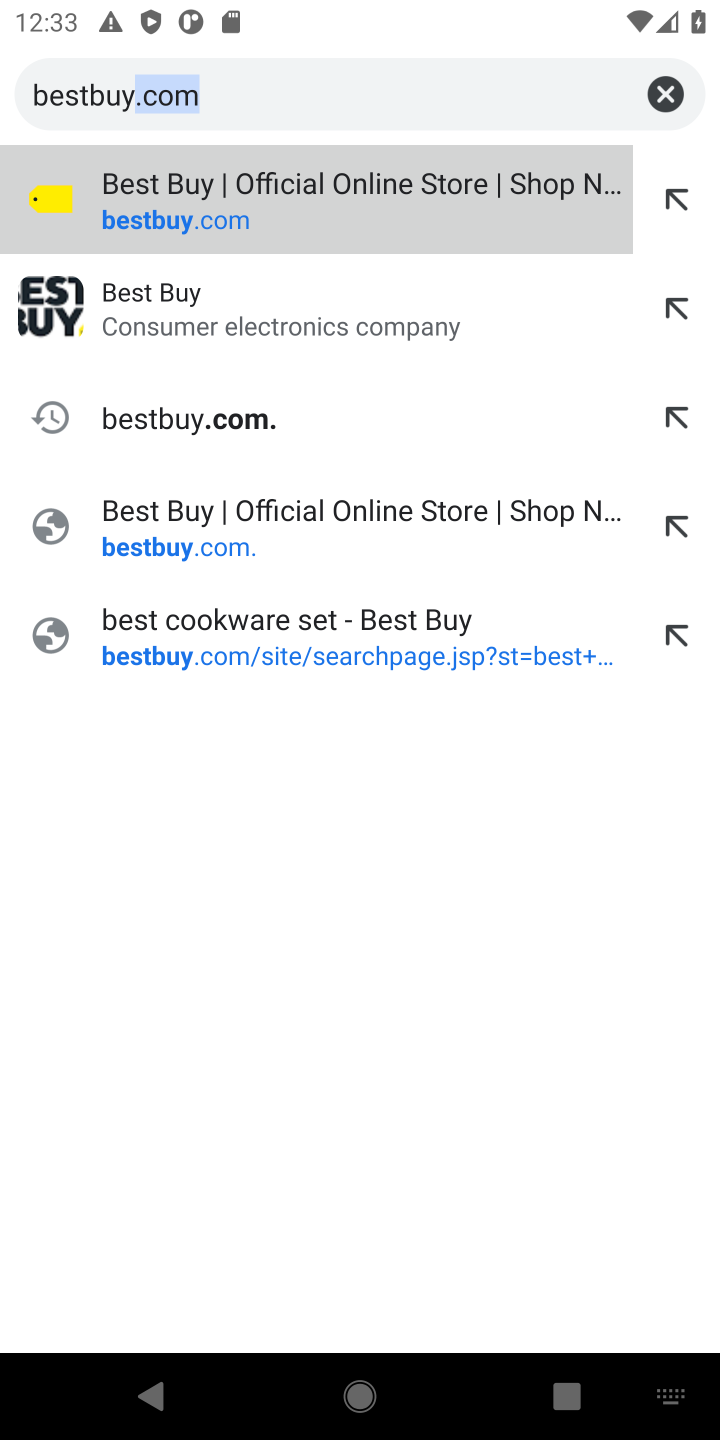
Step 32: click (229, 221)
Your task to perform on an android device: Add "razer blade" to the cart on bestbuy, then select checkout. Image 33: 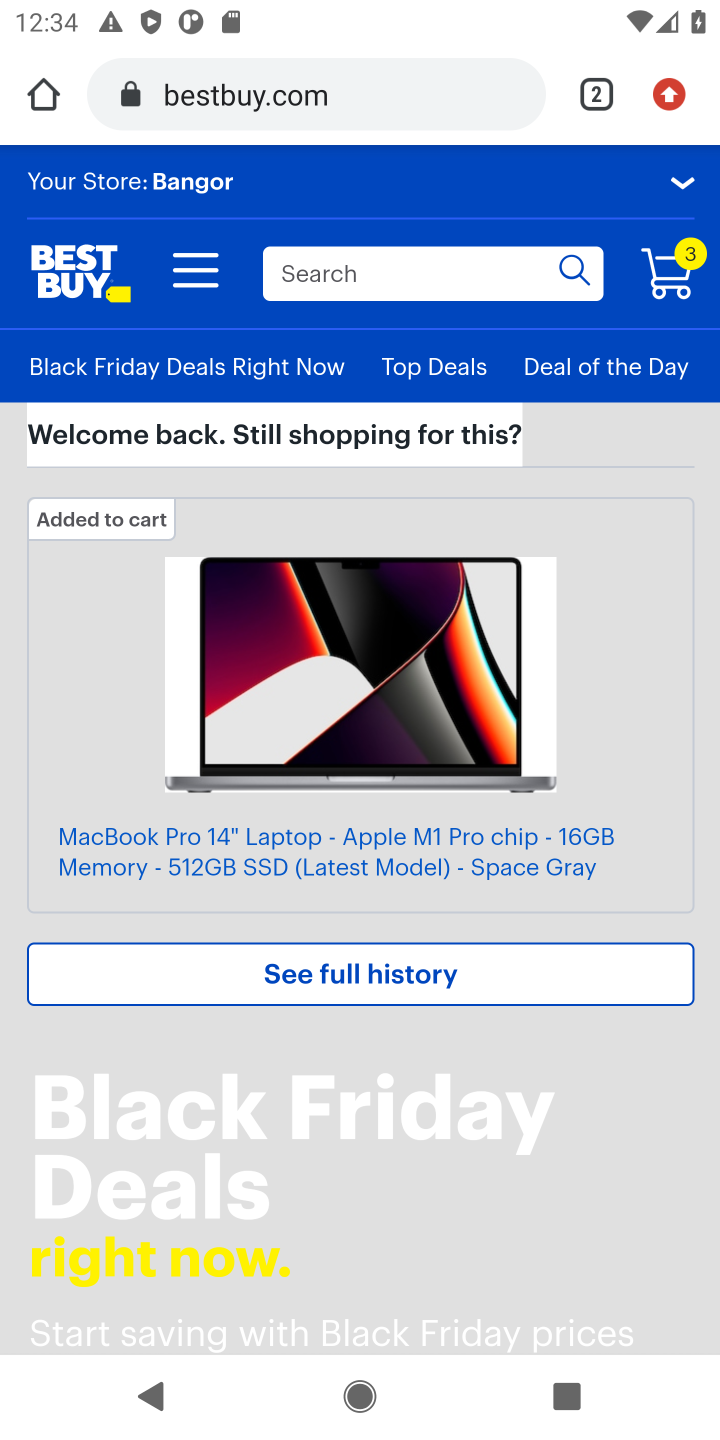
Step 33: click (382, 270)
Your task to perform on an android device: Add "razer blade" to the cart on bestbuy, then select checkout. Image 34: 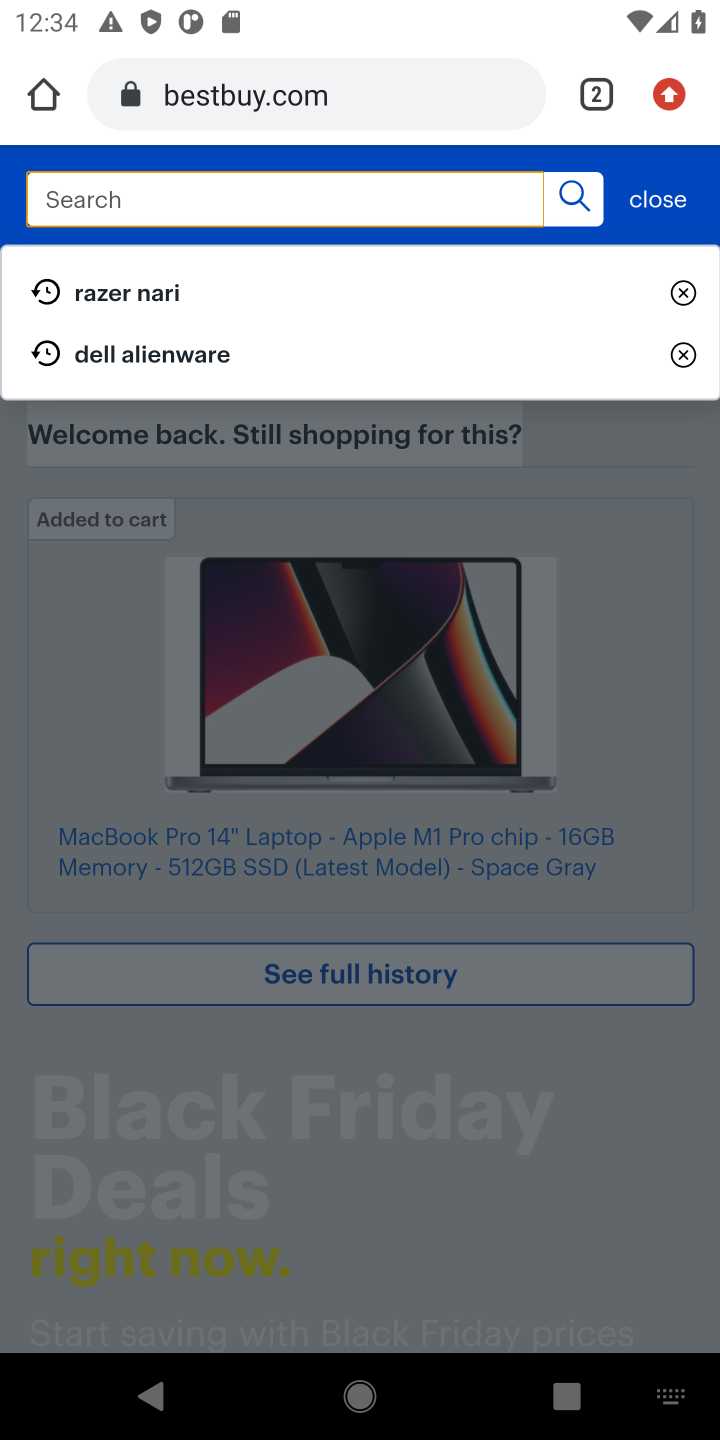
Step 34: type "razer blade"
Your task to perform on an android device: Add "razer blade" to the cart on bestbuy, then select checkout. Image 35: 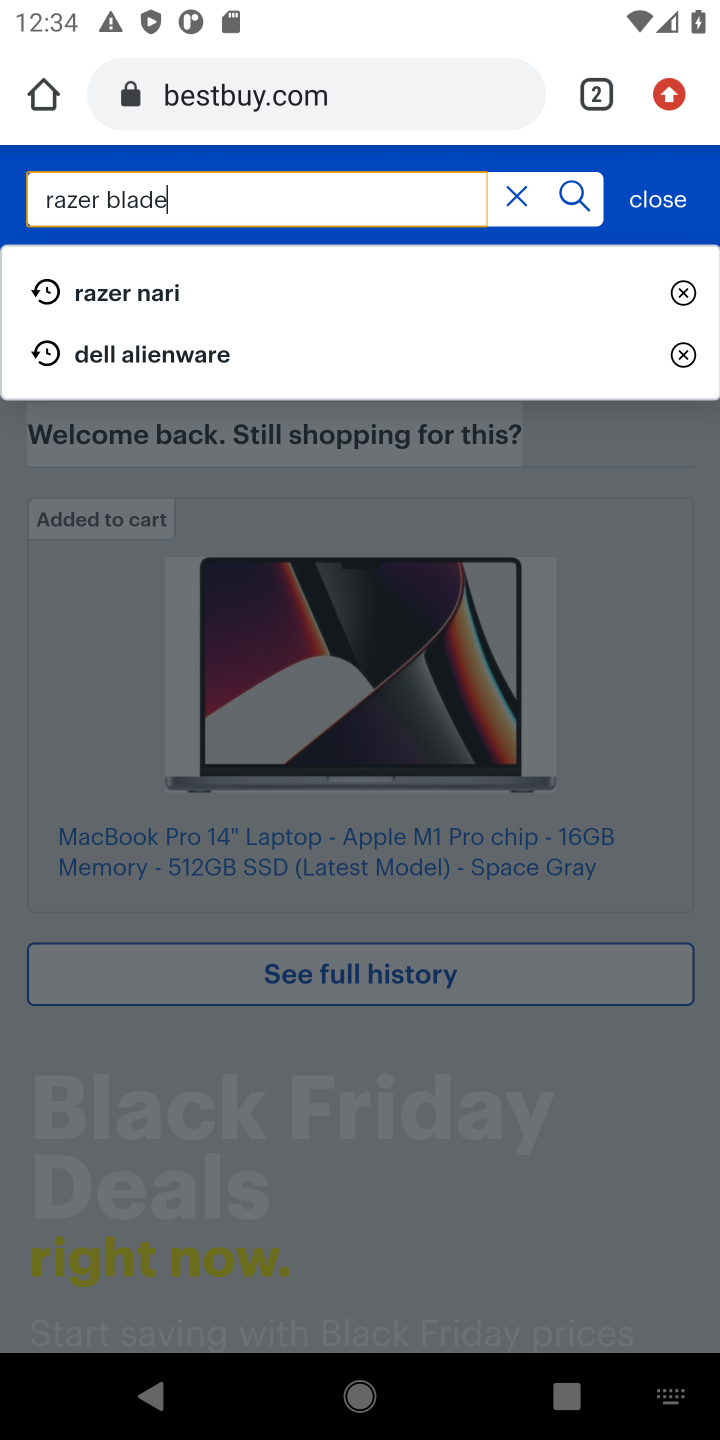
Step 35: type ""
Your task to perform on an android device: Add "razer blade" to the cart on bestbuy, then select checkout. Image 36: 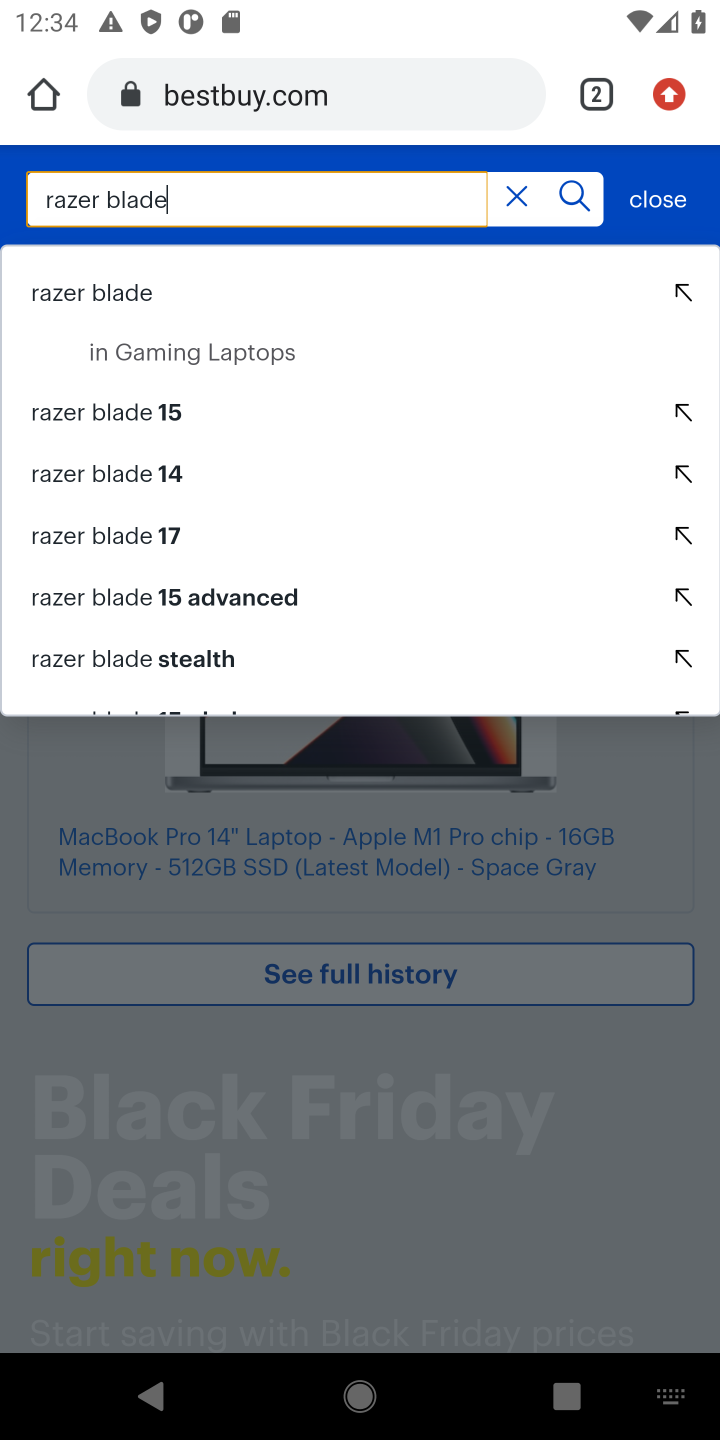
Step 36: click (156, 413)
Your task to perform on an android device: Add "razer blade" to the cart on bestbuy, then select checkout. Image 37: 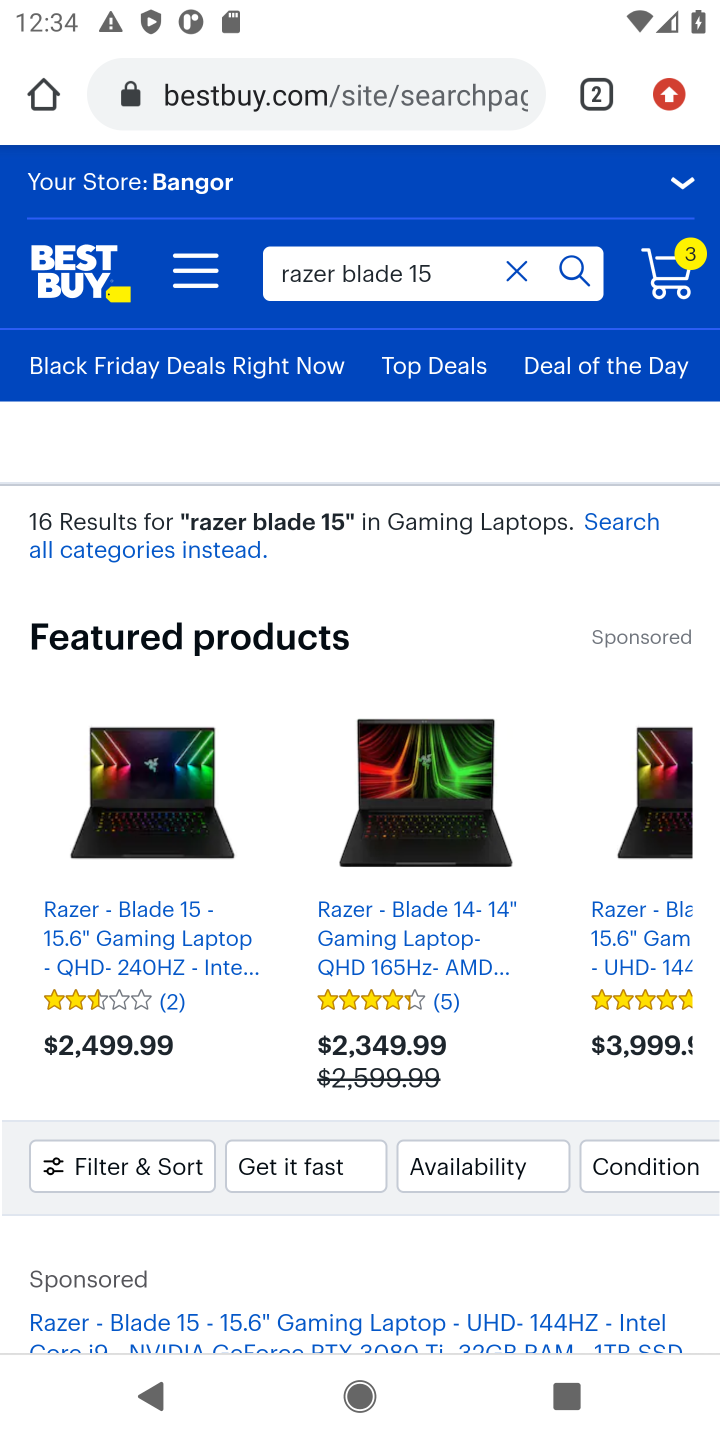
Step 37: click (186, 912)
Your task to perform on an android device: Add "razer blade" to the cart on bestbuy, then select checkout. Image 38: 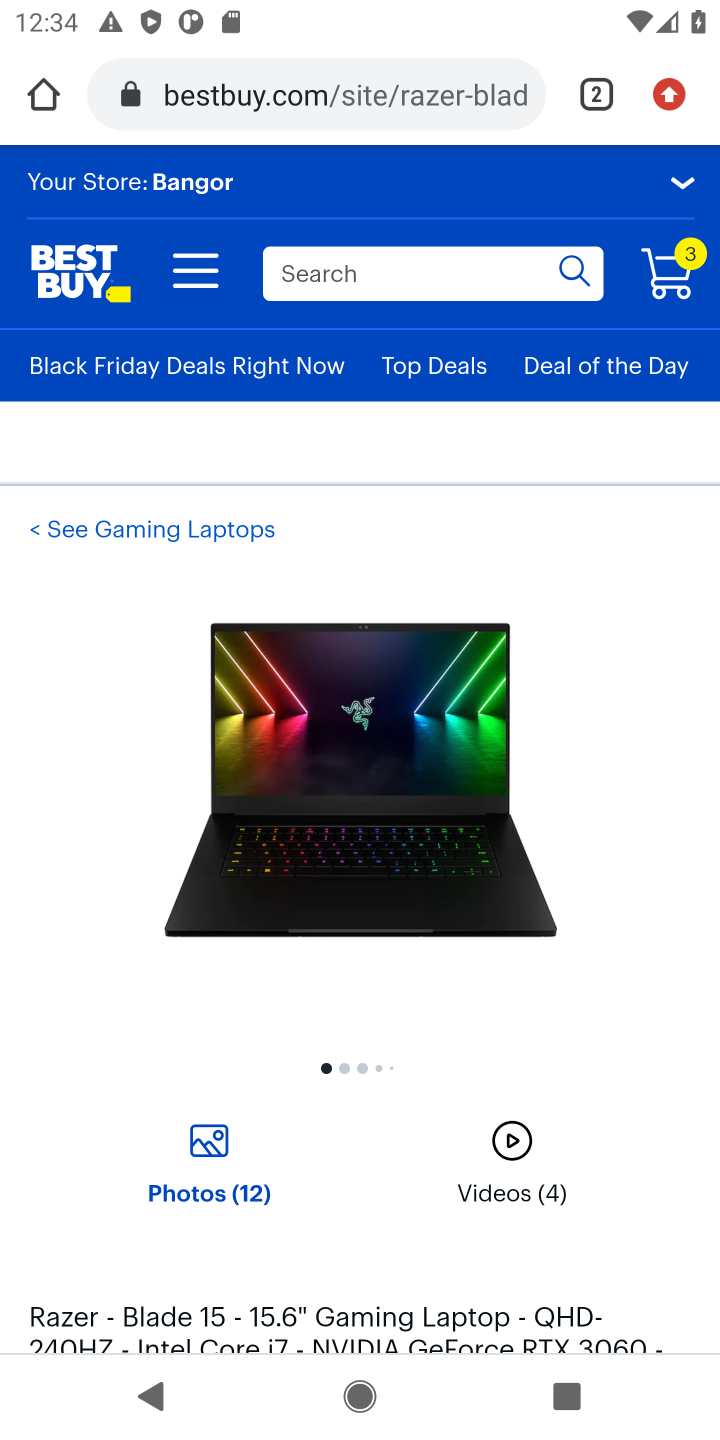
Step 38: drag from (280, 891) to (334, 513)
Your task to perform on an android device: Add "razer blade" to the cart on bestbuy, then select checkout. Image 39: 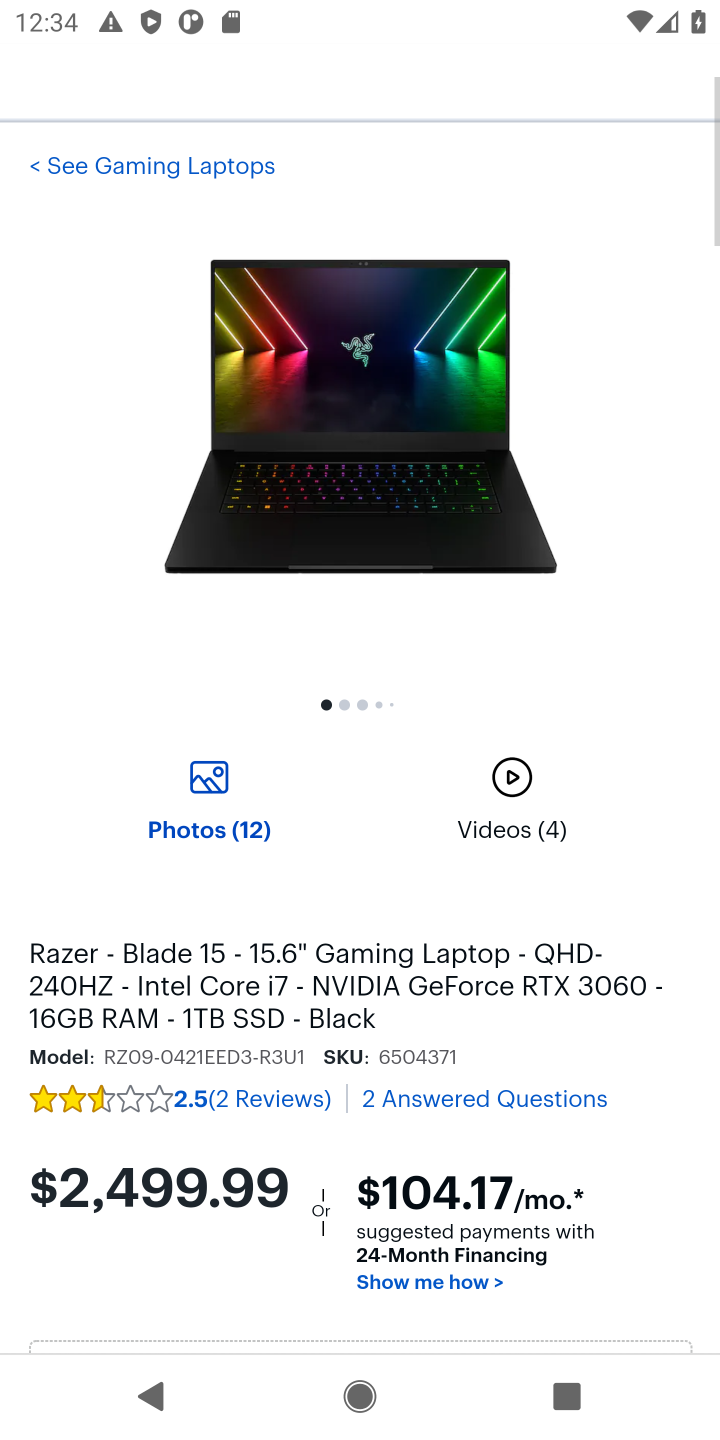
Step 39: drag from (370, 882) to (399, 517)
Your task to perform on an android device: Add "razer blade" to the cart on bestbuy, then select checkout. Image 40: 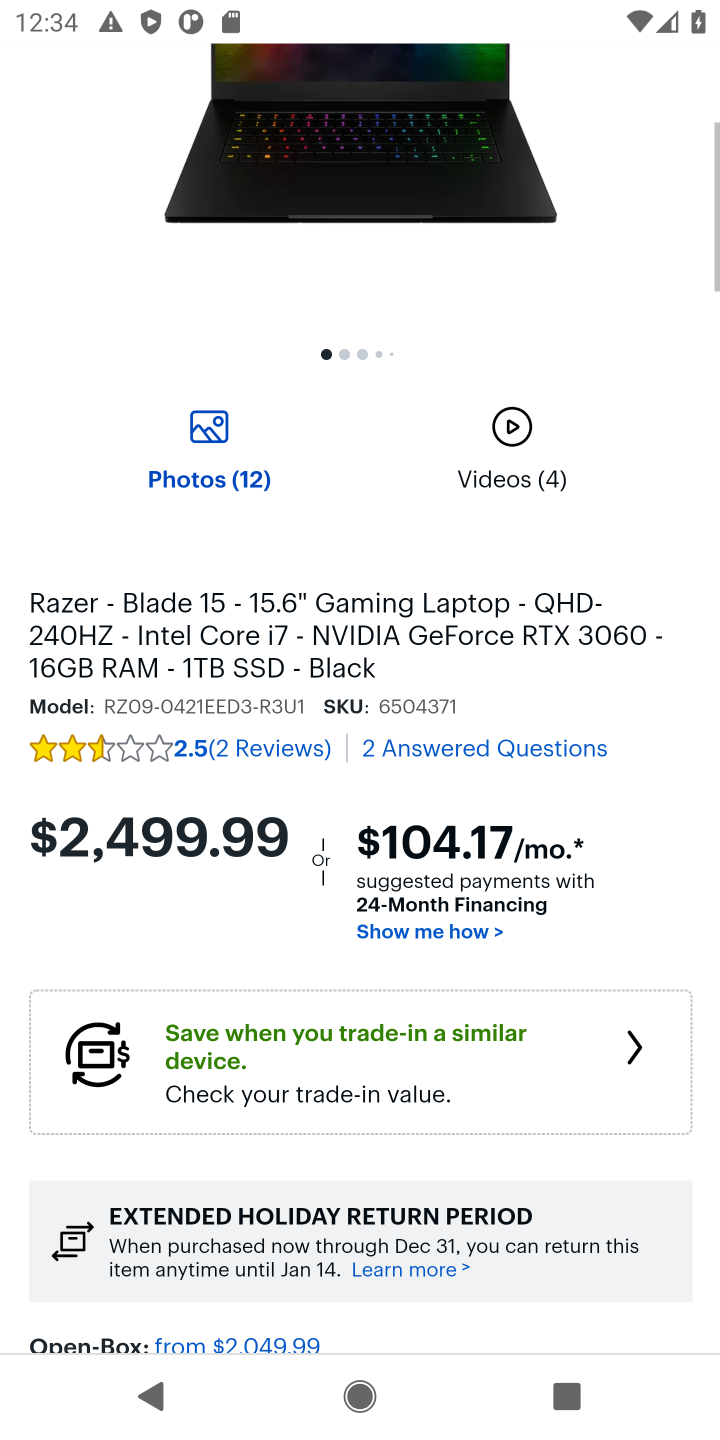
Step 40: drag from (457, 925) to (486, 591)
Your task to perform on an android device: Add "razer blade" to the cart on bestbuy, then select checkout. Image 41: 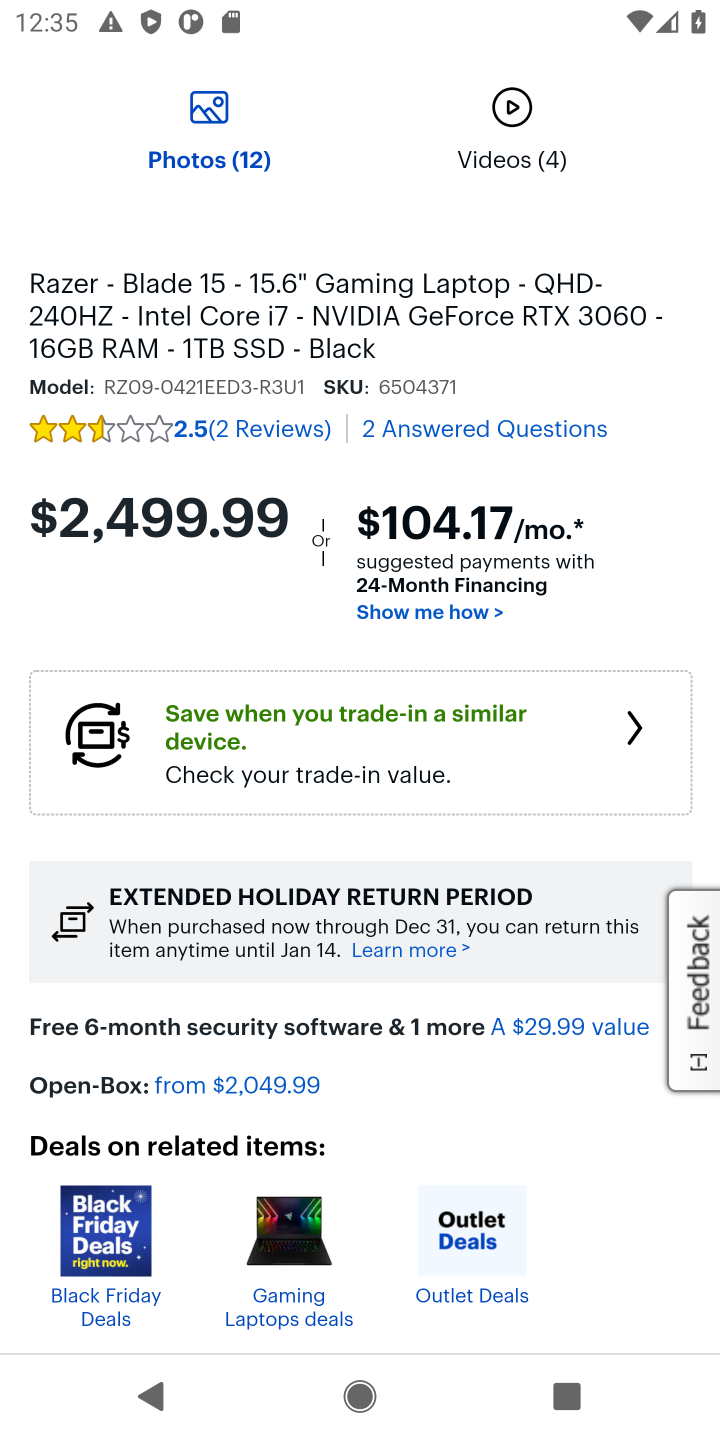
Step 41: click (460, 604)
Your task to perform on an android device: Add "razer blade" to the cart on bestbuy, then select checkout. Image 42: 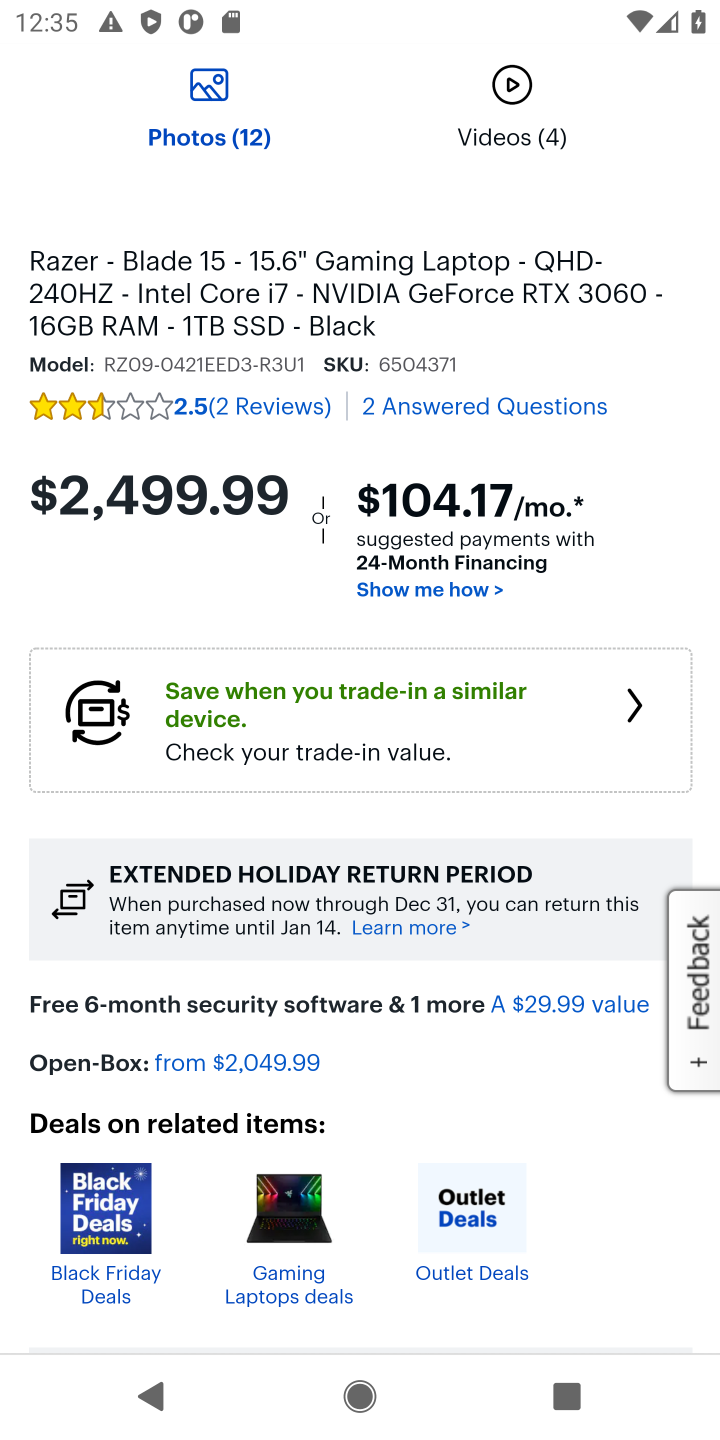
Step 42: drag from (403, 667) to (467, 439)
Your task to perform on an android device: Add "razer blade" to the cart on bestbuy, then select checkout. Image 43: 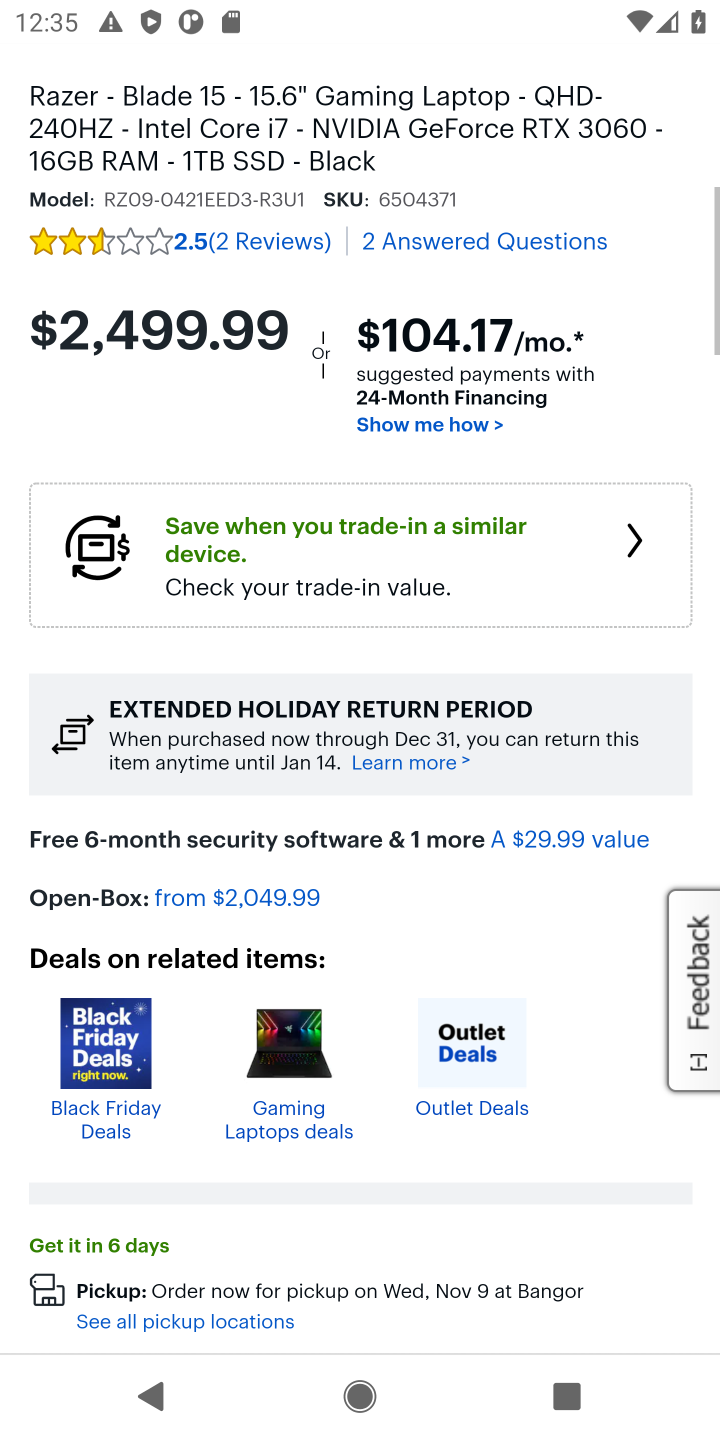
Step 43: drag from (397, 574) to (463, 324)
Your task to perform on an android device: Add "razer blade" to the cart on bestbuy, then select checkout. Image 44: 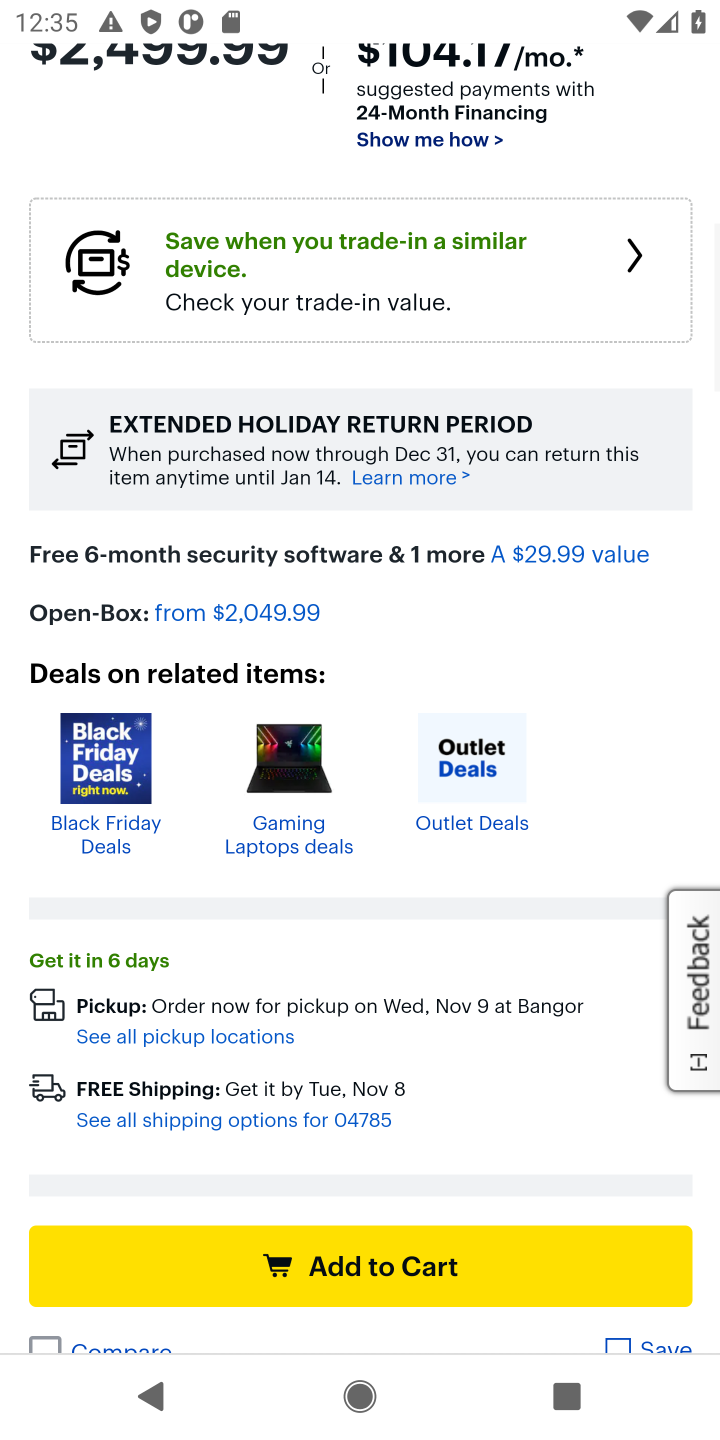
Step 44: click (494, 334)
Your task to perform on an android device: Add "razer blade" to the cart on bestbuy, then select checkout. Image 45: 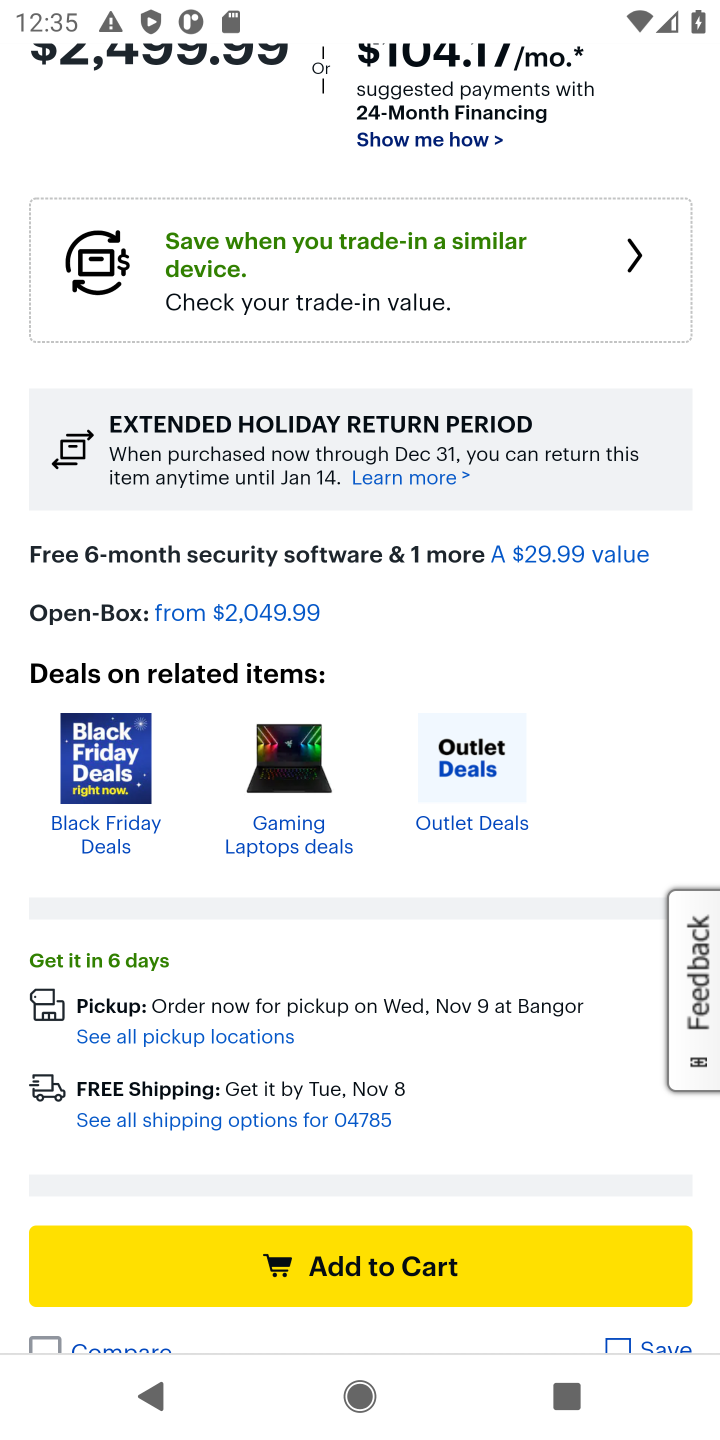
Step 45: drag from (519, 790) to (428, 344)
Your task to perform on an android device: Add "razer blade" to the cart on bestbuy, then select checkout. Image 46: 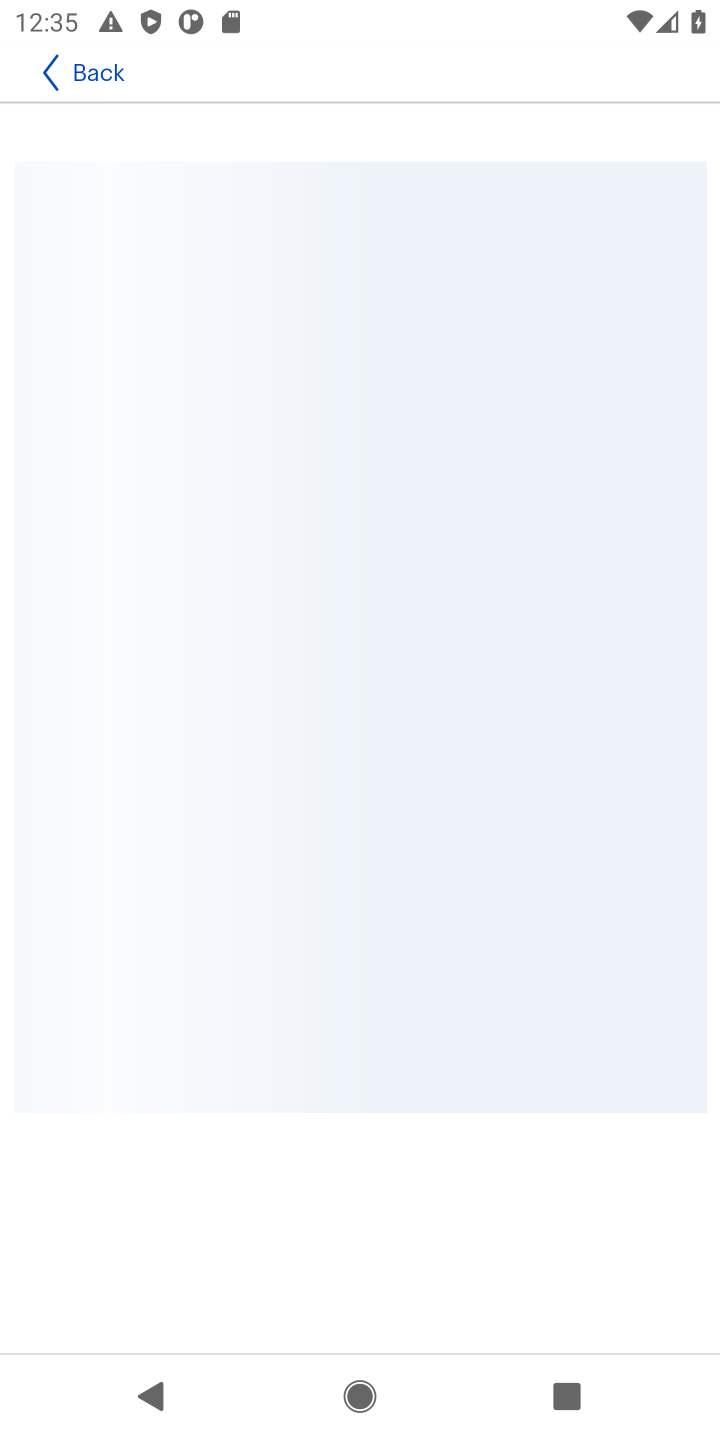
Step 46: drag from (423, 1023) to (459, 438)
Your task to perform on an android device: Add "razer blade" to the cart on bestbuy, then select checkout. Image 47: 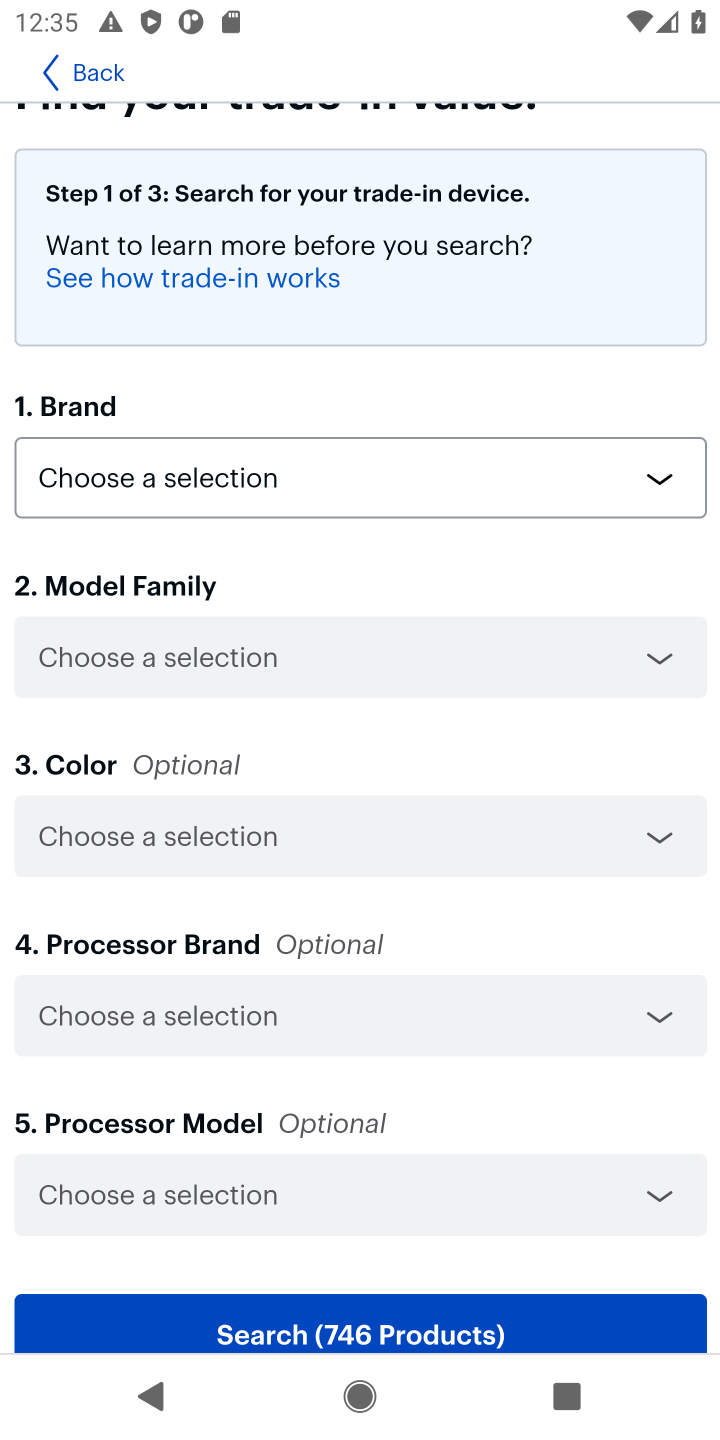
Step 47: click (80, 62)
Your task to perform on an android device: Add "razer blade" to the cart on bestbuy, then select checkout. Image 48: 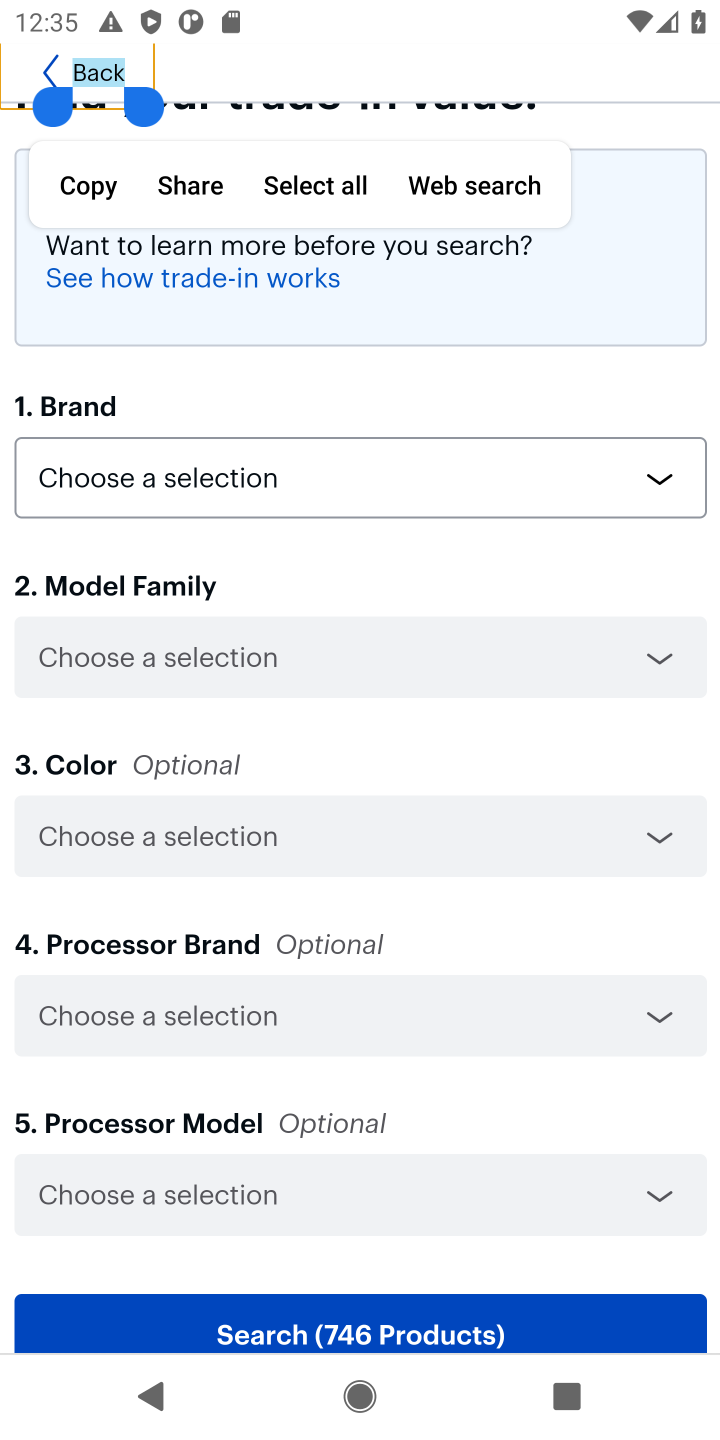
Step 48: click (56, 60)
Your task to perform on an android device: Add "razer blade" to the cart on bestbuy, then select checkout. Image 49: 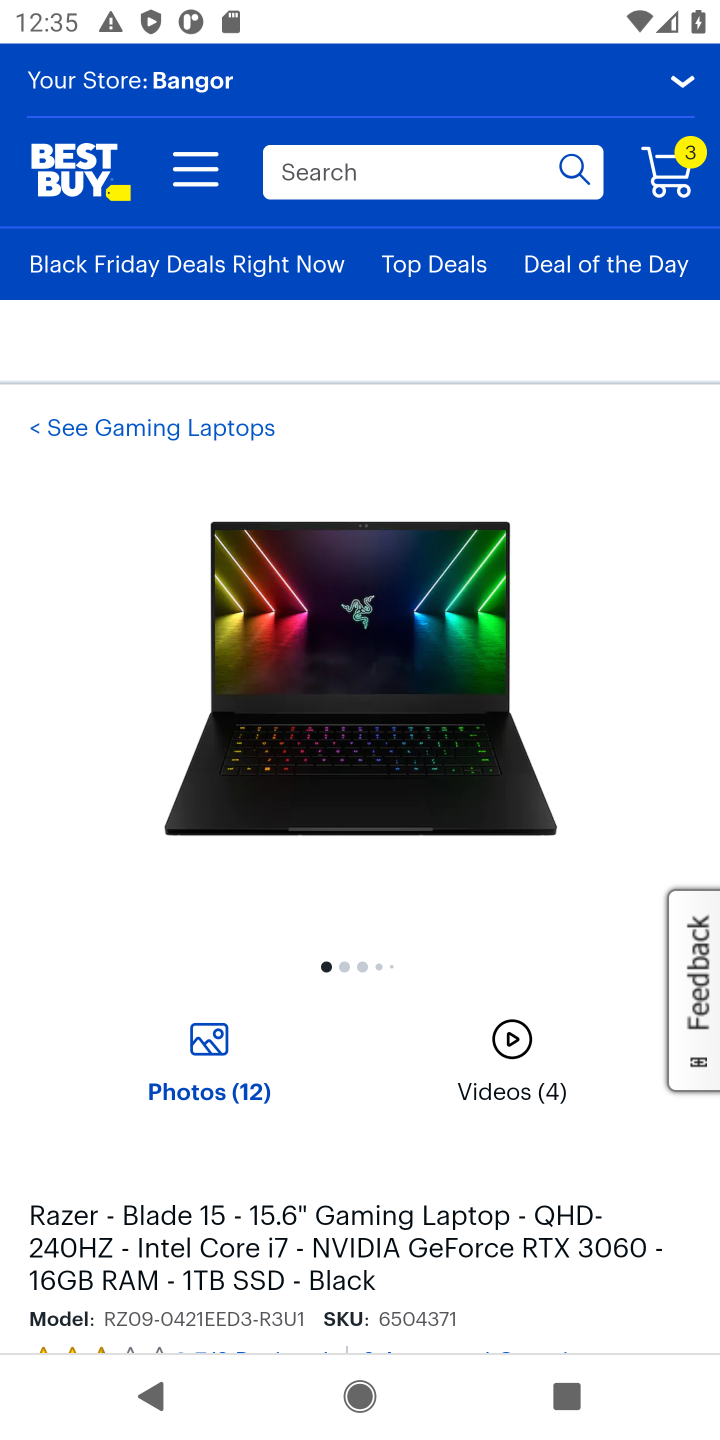
Step 49: drag from (366, 1226) to (417, 488)
Your task to perform on an android device: Add "razer blade" to the cart on bestbuy, then select checkout. Image 50: 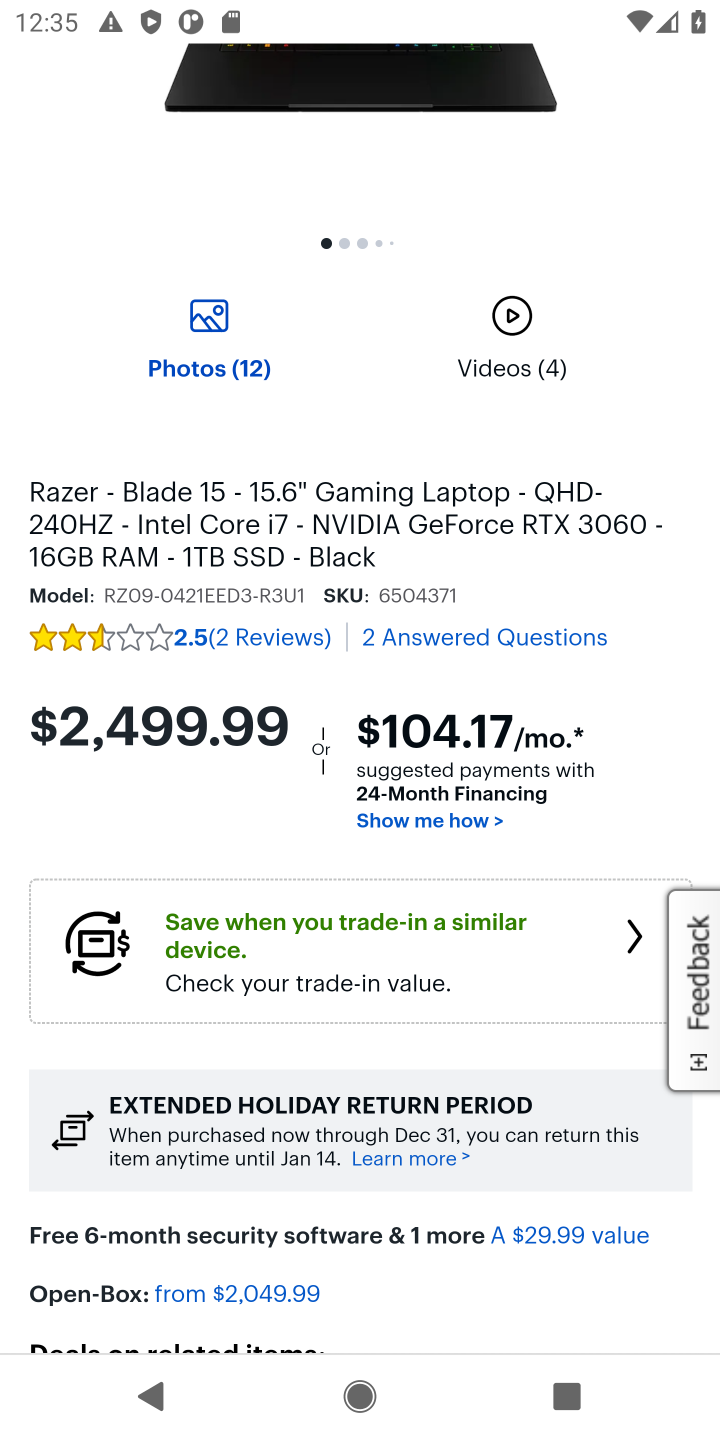
Step 50: drag from (361, 1123) to (461, 458)
Your task to perform on an android device: Add "razer blade" to the cart on bestbuy, then select checkout. Image 51: 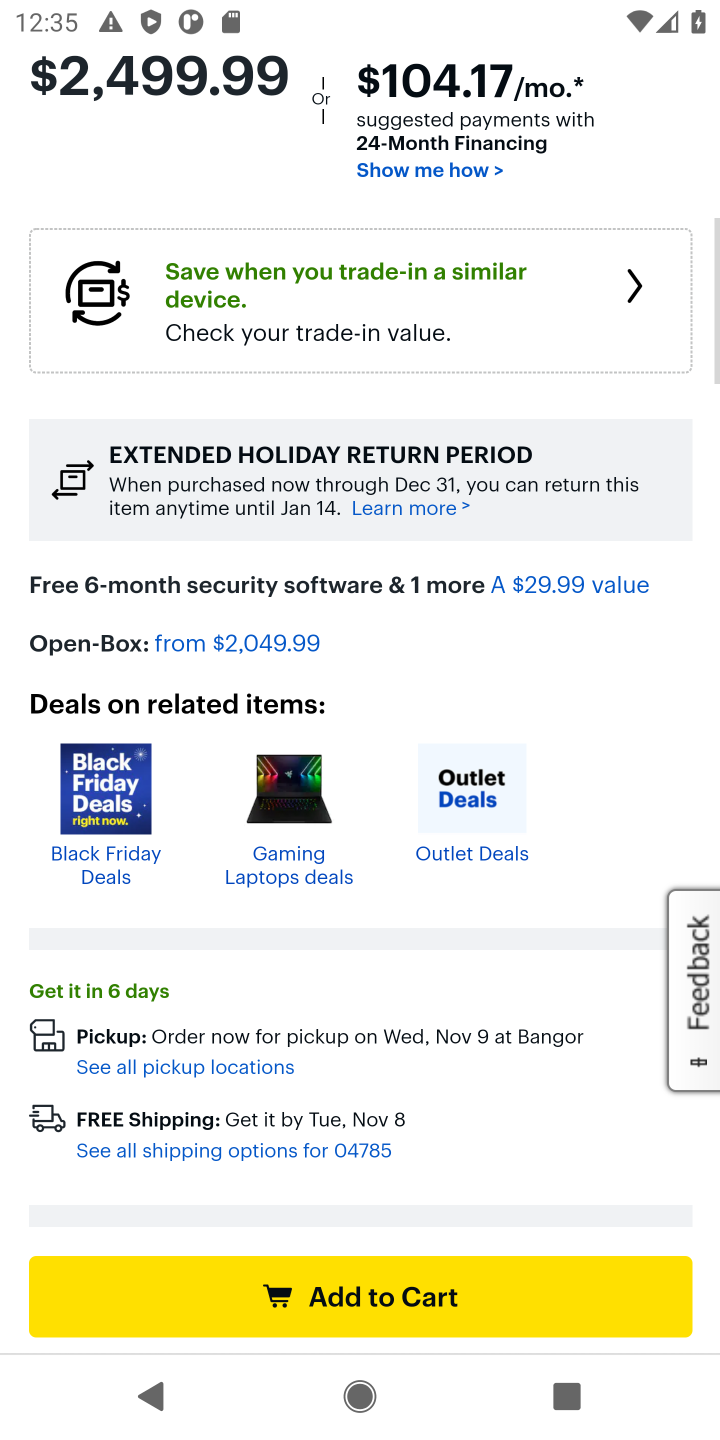
Step 51: click (397, 1301)
Your task to perform on an android device: Add "razer blade" to the cart on bestbuy, then select checkout. Image 52: 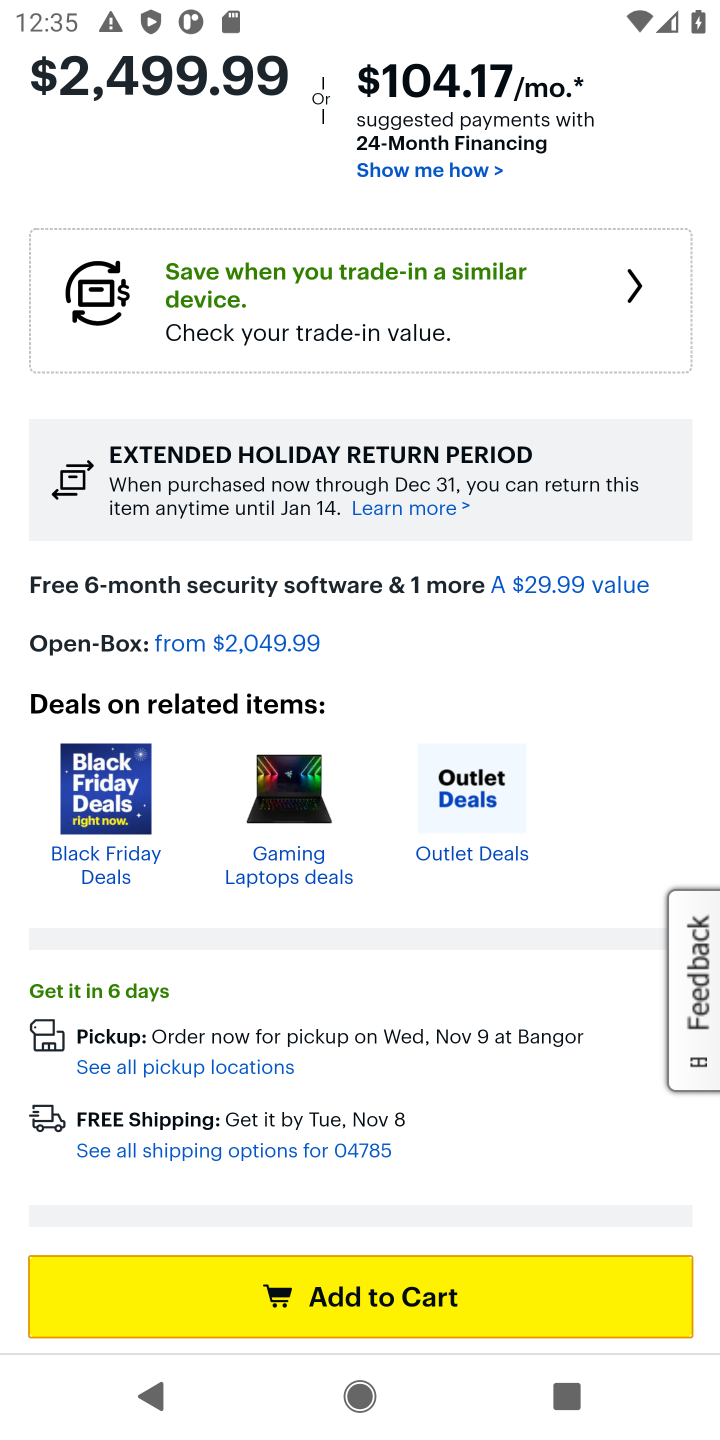
Step 52: click (397, 1301)
Your task to perform on an android device: Add "razer blade" to the cart on bestbuy, then select checkout. Image 53: 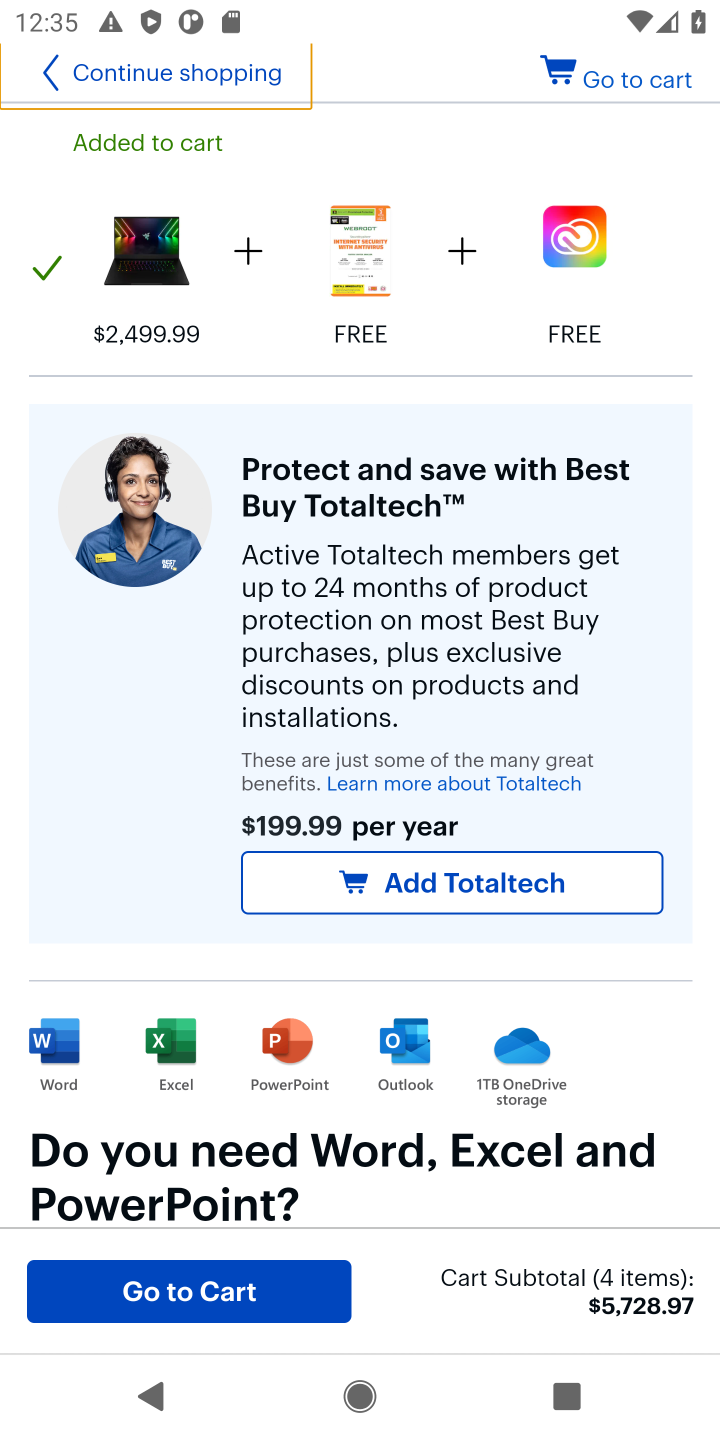
Step 53: click (608, 82)
Your task to perform on an android device: Add "razer blade" to the cart on bestbuy, then select checkout. Image 54: 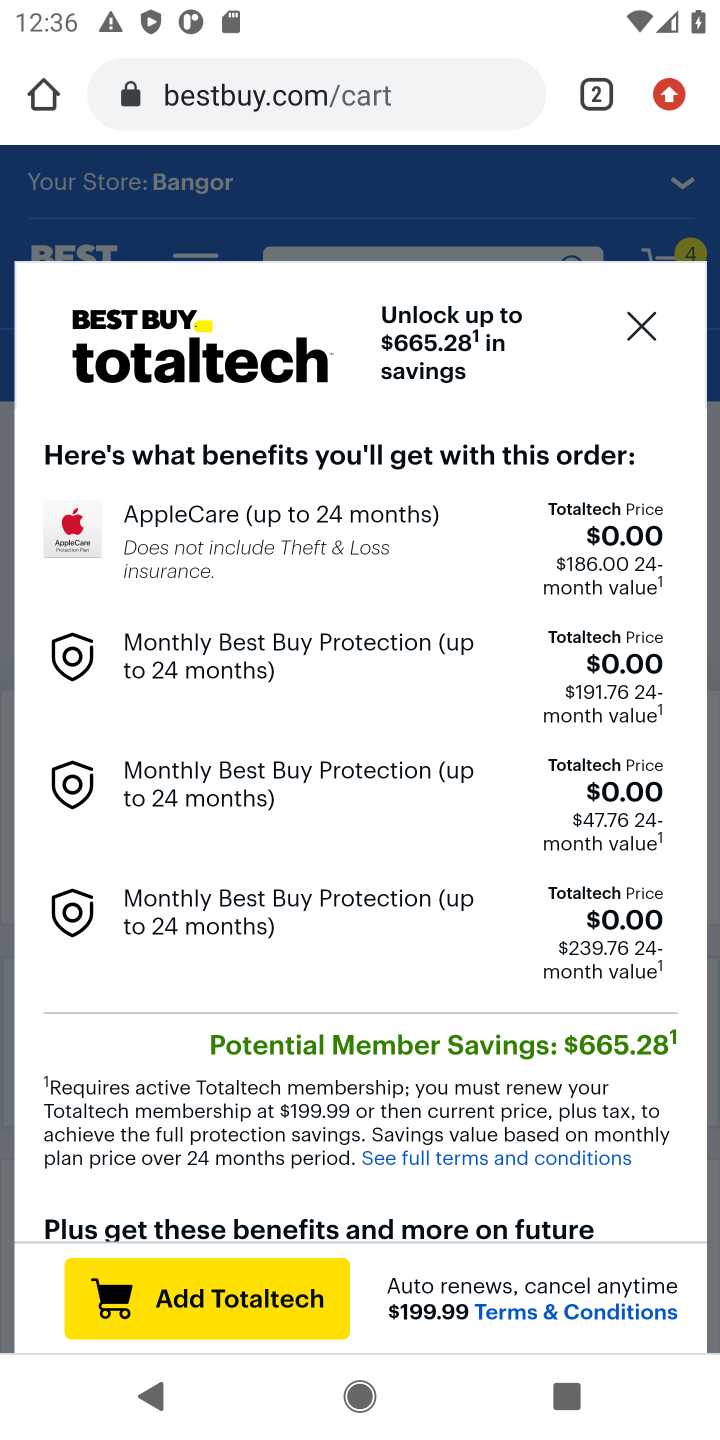
Step 54: click (654, 330)
Your task to perform on an android device: Add "razer blade" to the cart on bestbuy, then select checkout. Image 55: 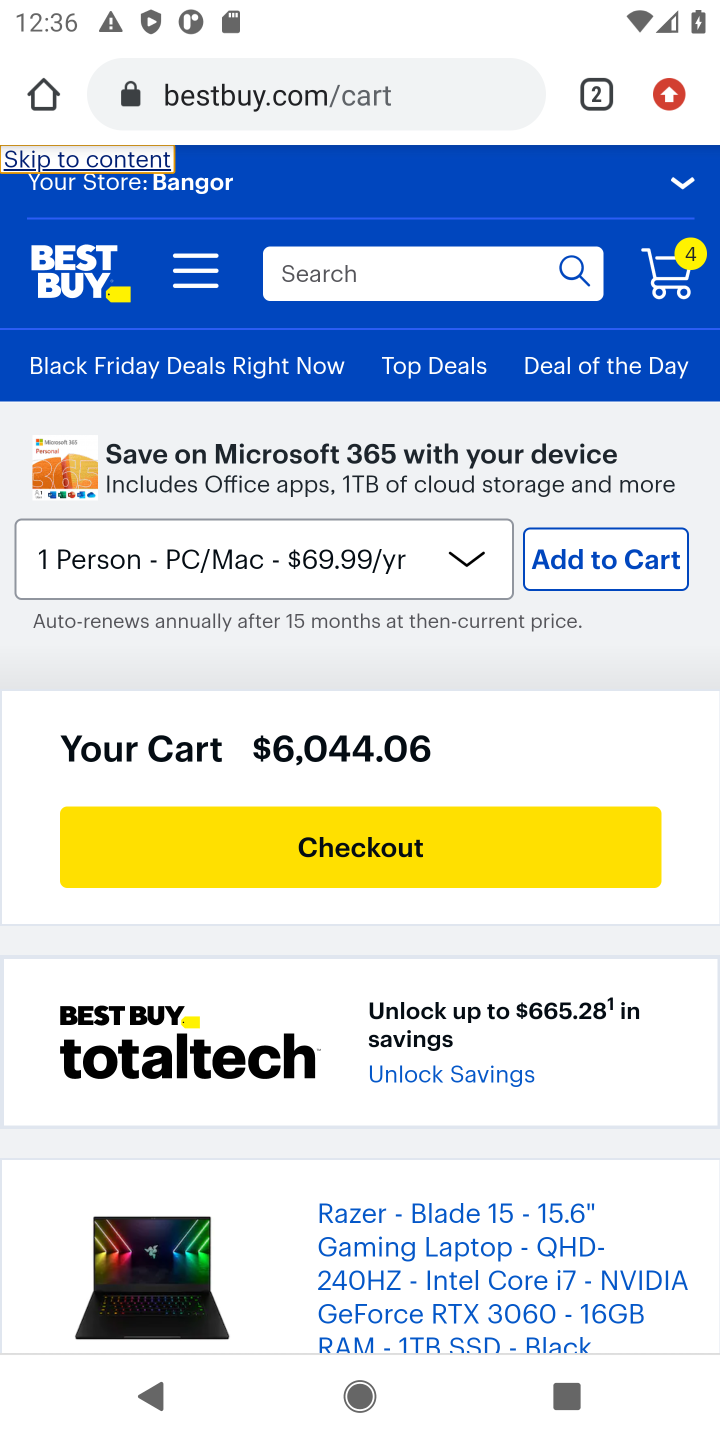
Step 55: drag from (485, 1138) to (592, 421)
Your task to perform on an android device: Add "razer blade" to the cart on bestbuy, then select checkout. Image 56: 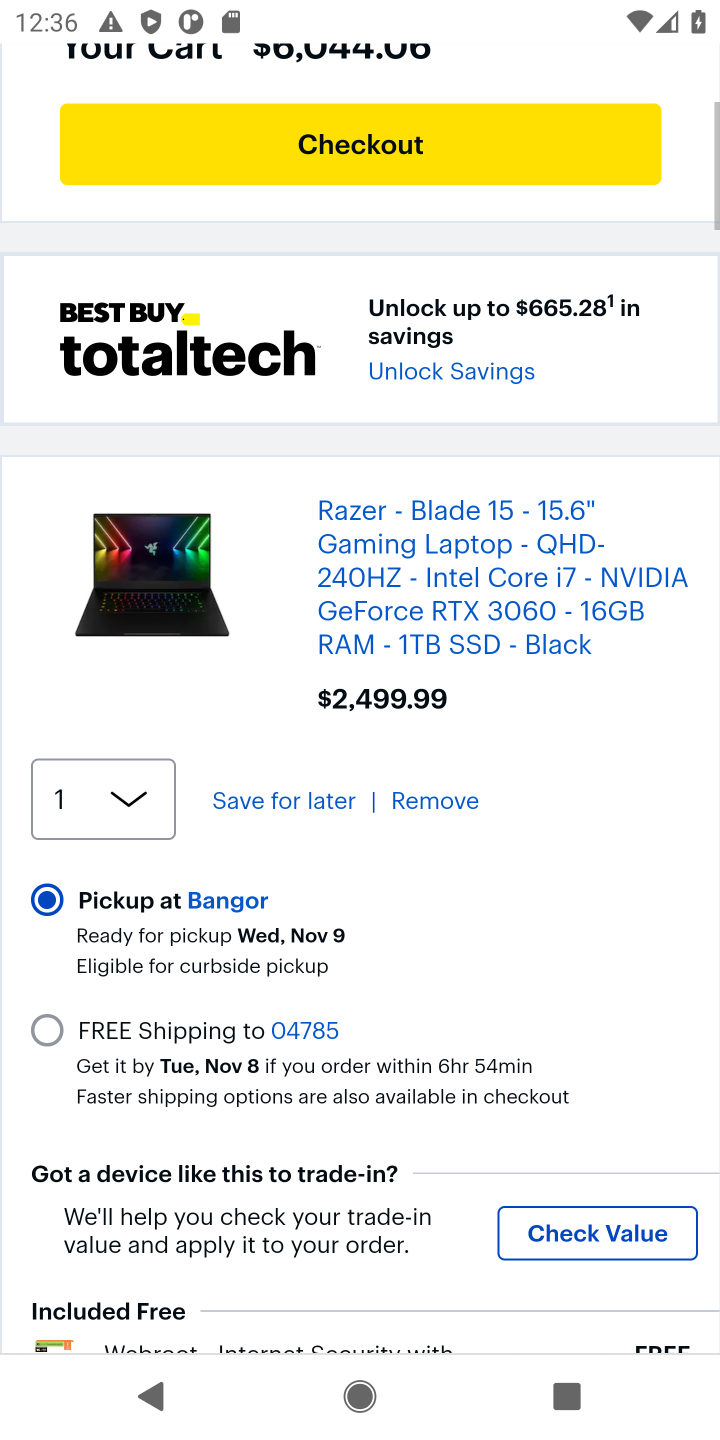
Step 56: drag from (423, 1265) to (572, 442)
Your task to perform on an android device: Add "razer blade" to the cart on bestbuy, then select checkout. Image 57: 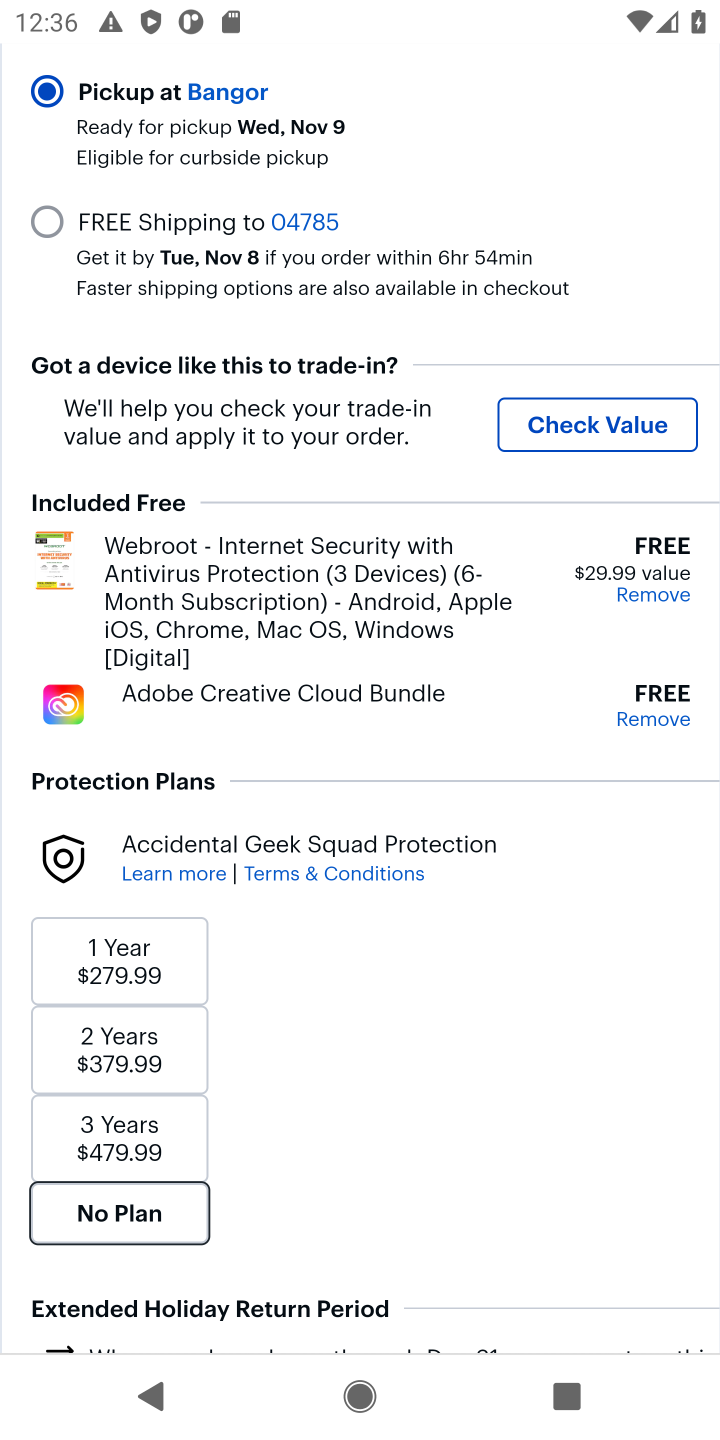
Step 57: click (637, 598)
Your task to perform on an android device: Add "razer blade" to the cart on bestbuy, then select checkout. Image 58: 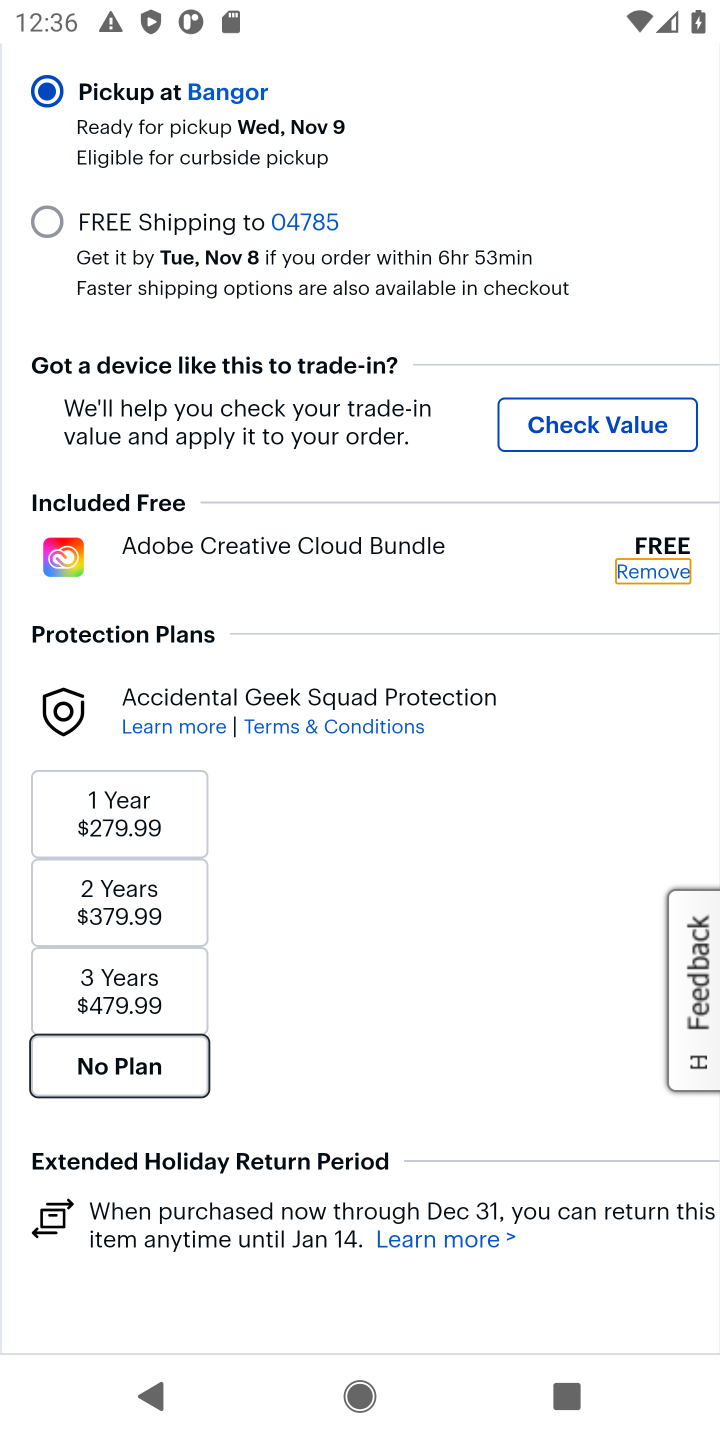
Step 58: click (641, 571)
Your task to perform on an android device: Add "razer blade" to the cart on bestbuy, then select checkout. Image 59: 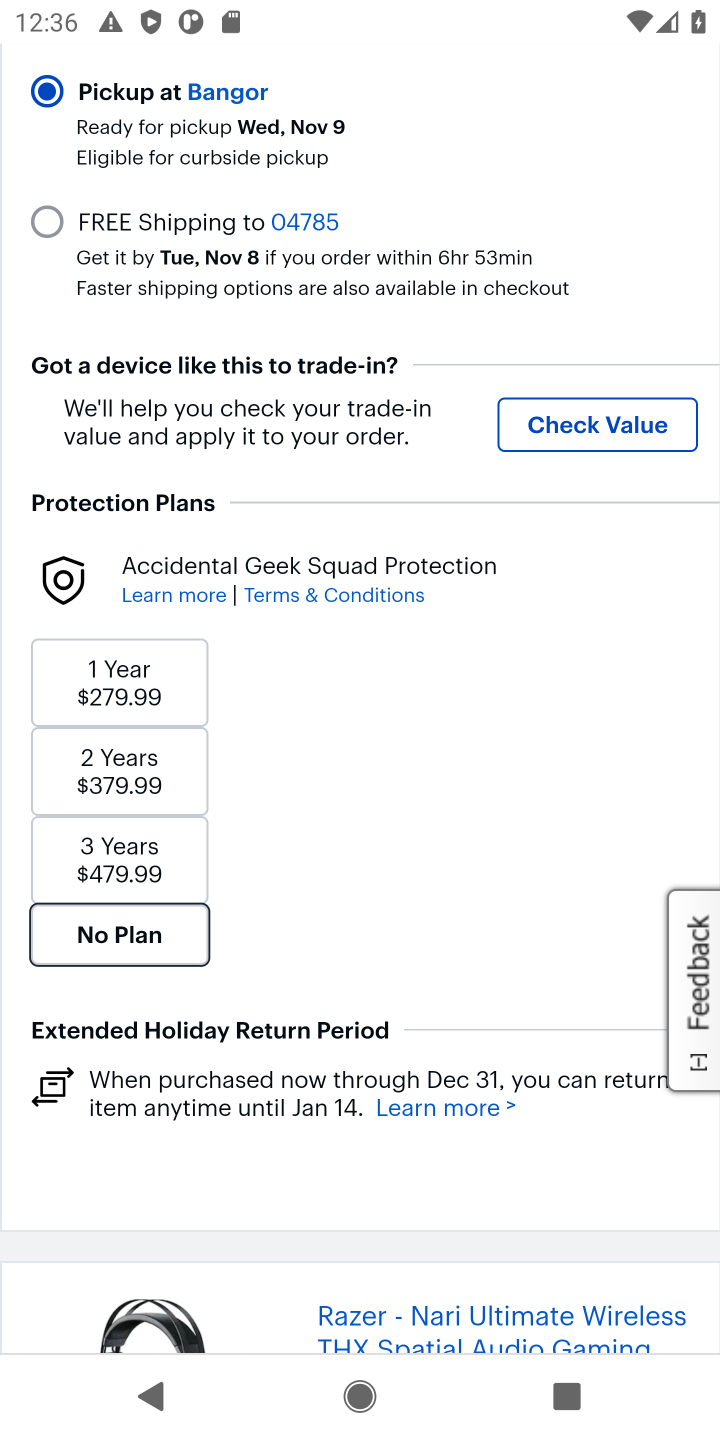
Step 59: drag from (466, 1066) to (526, 276)
Your task to perform on an android device: Add "razer blade" to the cart on bestbuy, then select checkout. Image 60: 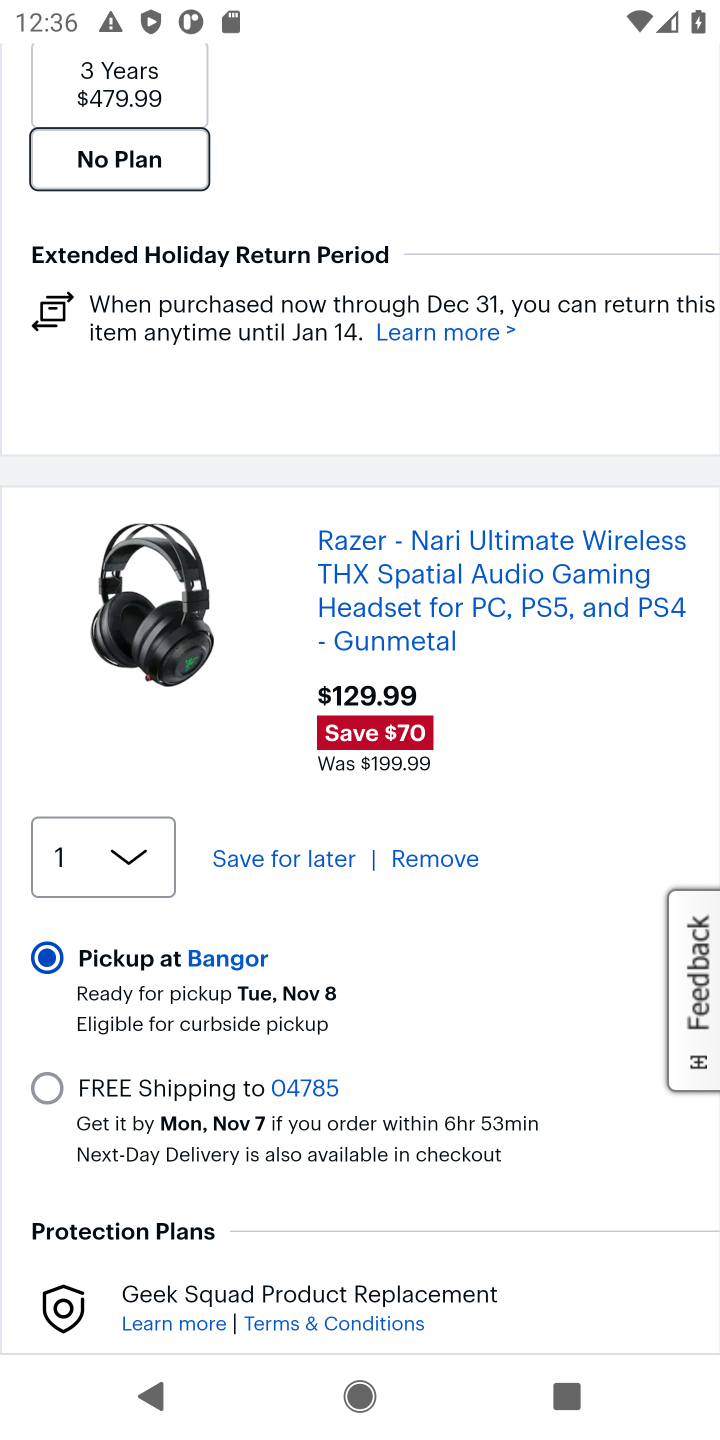
Step 60: click (434, 840)
Your task to perform on an android device: Add "razer blade" to the cart on bestbuy, then select checkout. Image 61: 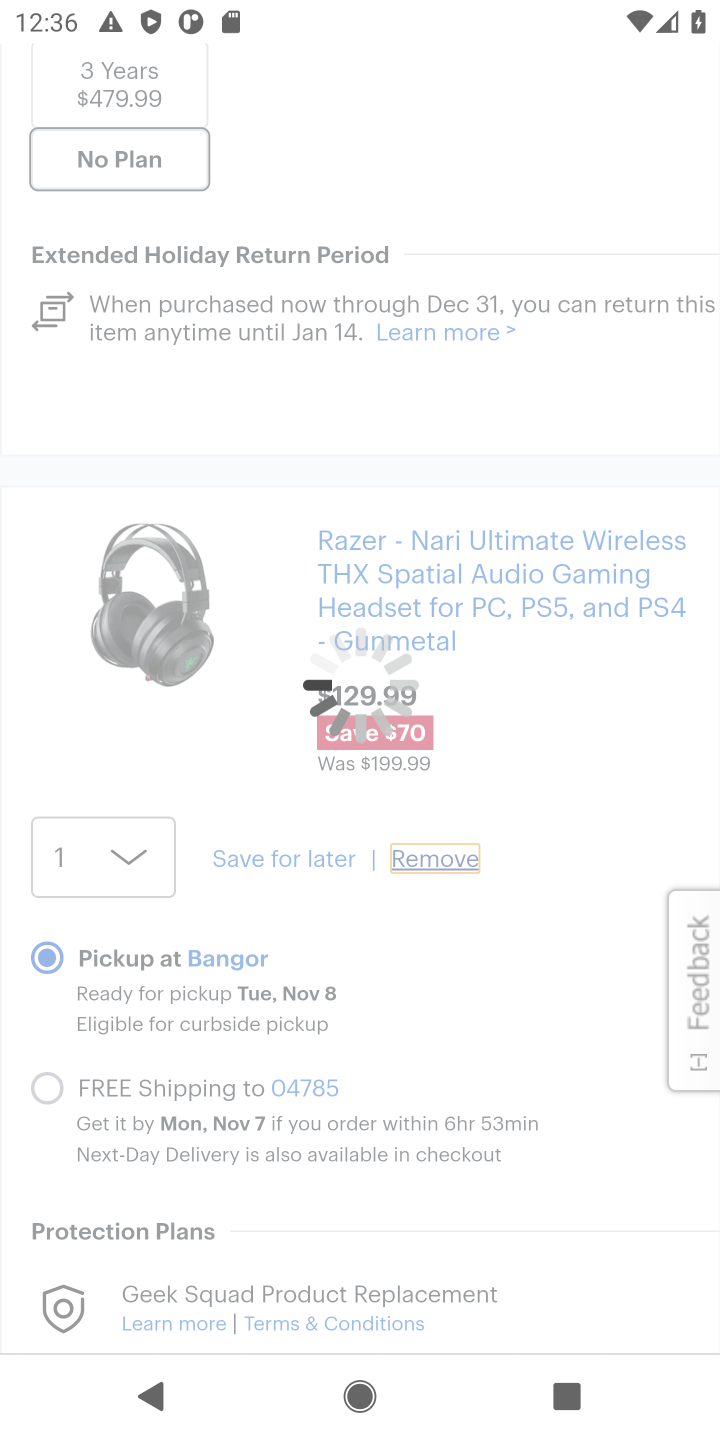
Step 61: click (430, 865)
Your task to perform on an android device: Add "razer blade" to the cart on bestbuy, then select checkout. Image 62: 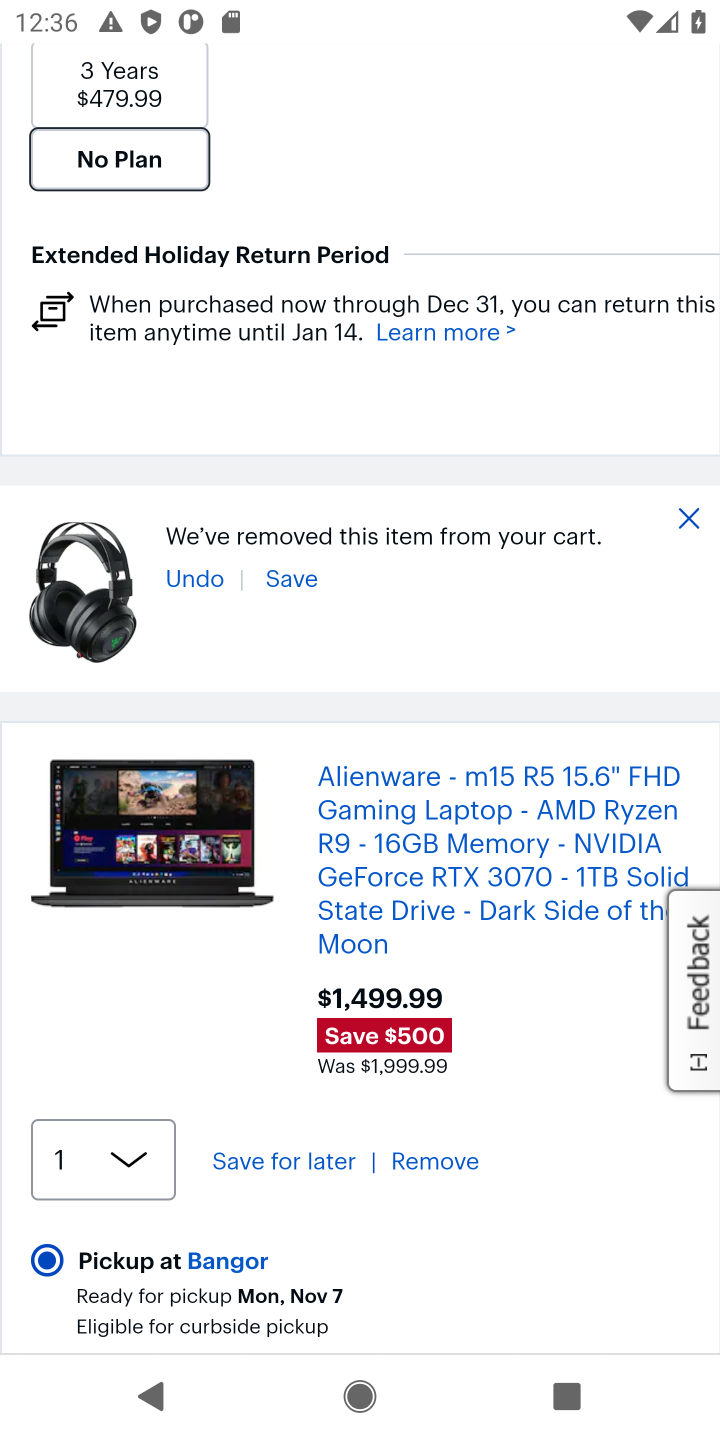
Step 62: drag from (504, 1054) to (566, 445)
Your task to perform on an android device: Add "razer blade" to the cart on bestbuy, then select checkout. Image 63: 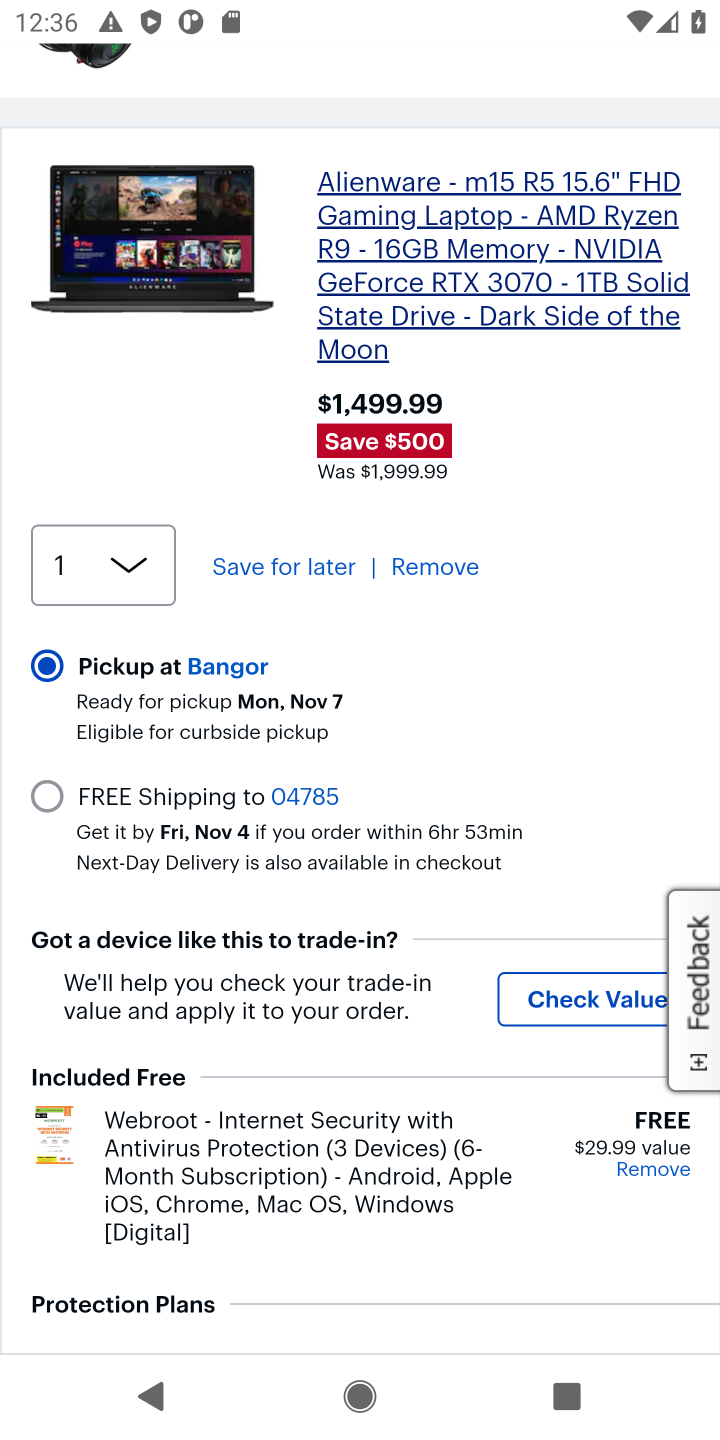
Step 63: drag from (539, 867) to (565, 648)
Your task to perform on an android device: Add "razer blade" to the cart on bestbuy, then select checkout. Image 64: 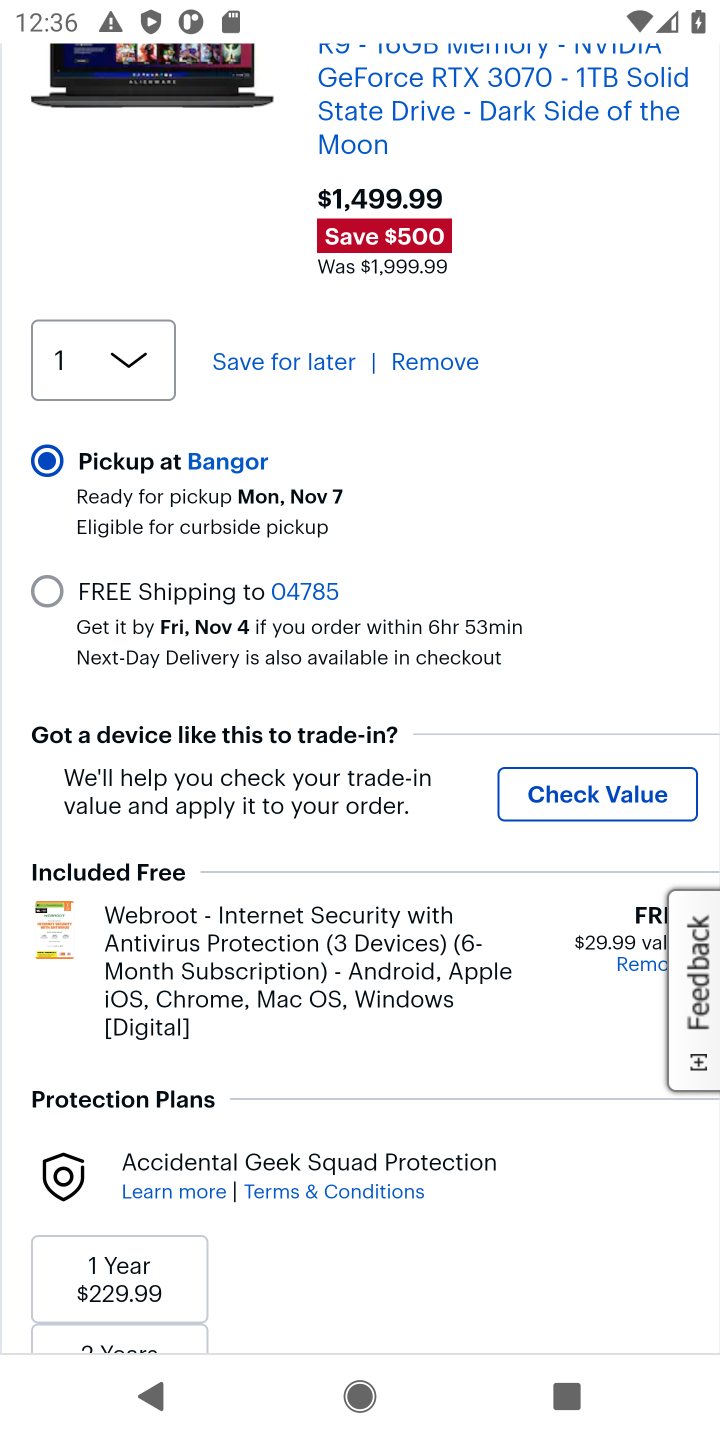
Step 64: click (637, 962)
Your task to perform on an android device: Add "razer blade" to the cart on bestbuy, then select checkout. Image 65: 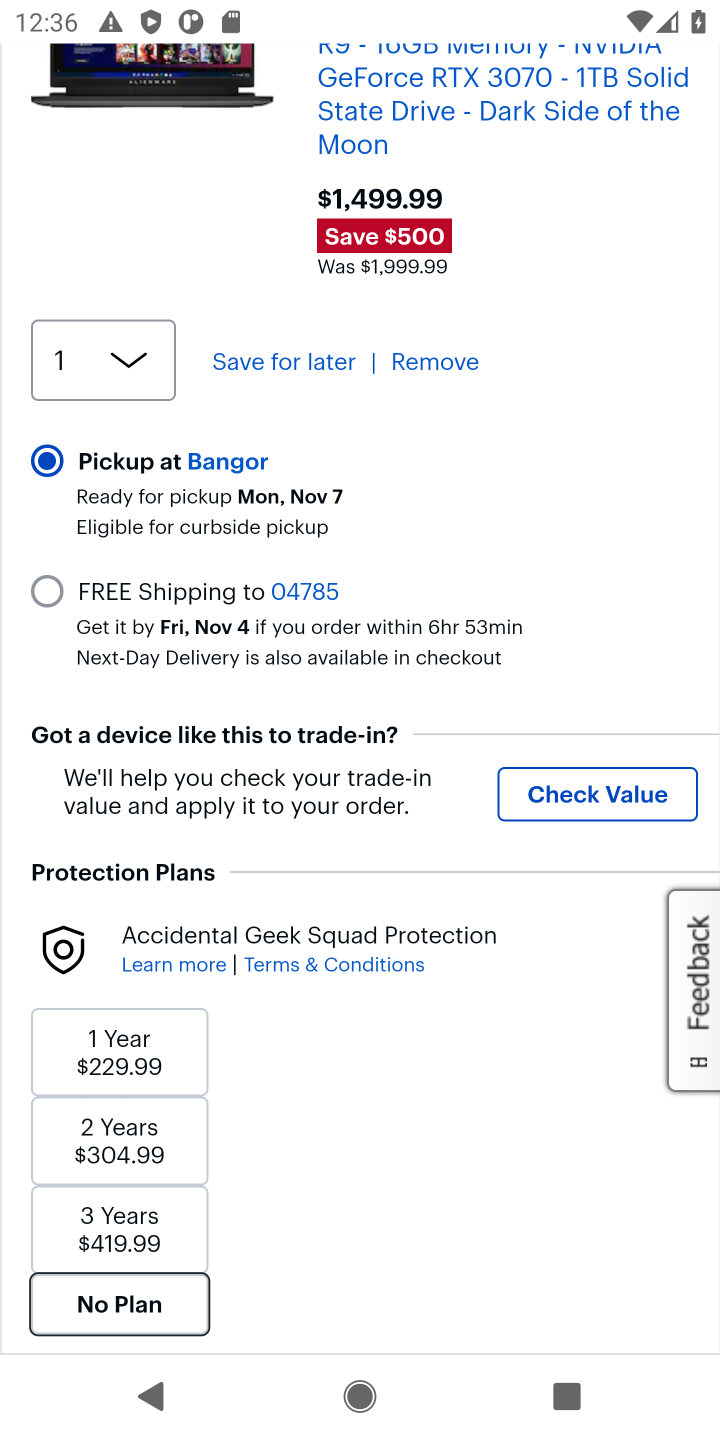
Step 65: drag from (500, 996) to (535, 494)
Your task to perform on an android device: Add "razer blade" to the cart on bestbuy, then select checkout. Image 66: 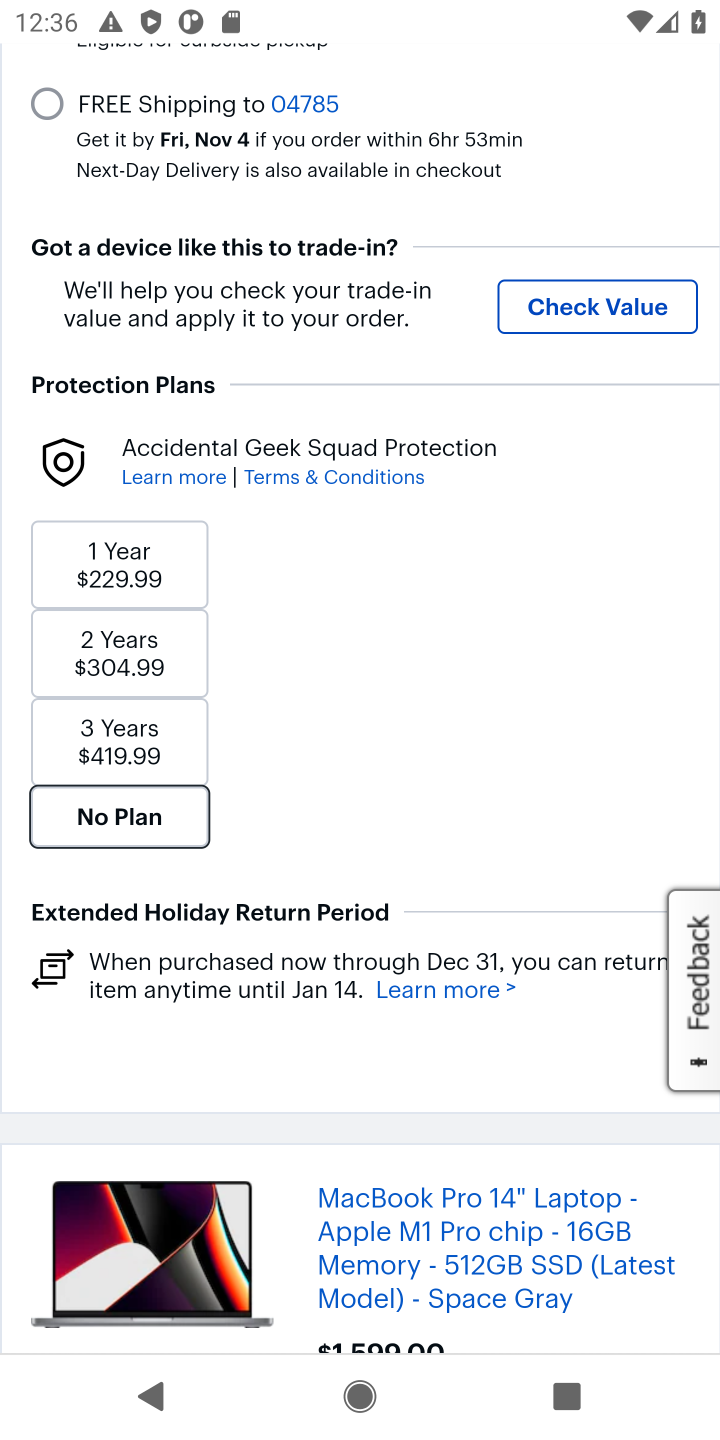
Step 66: drag from (398, 863) to (449, 576)
Your task to perform on an android device: Add "razer blade" to the cart on bestbuy, then select checkout. Image 67: 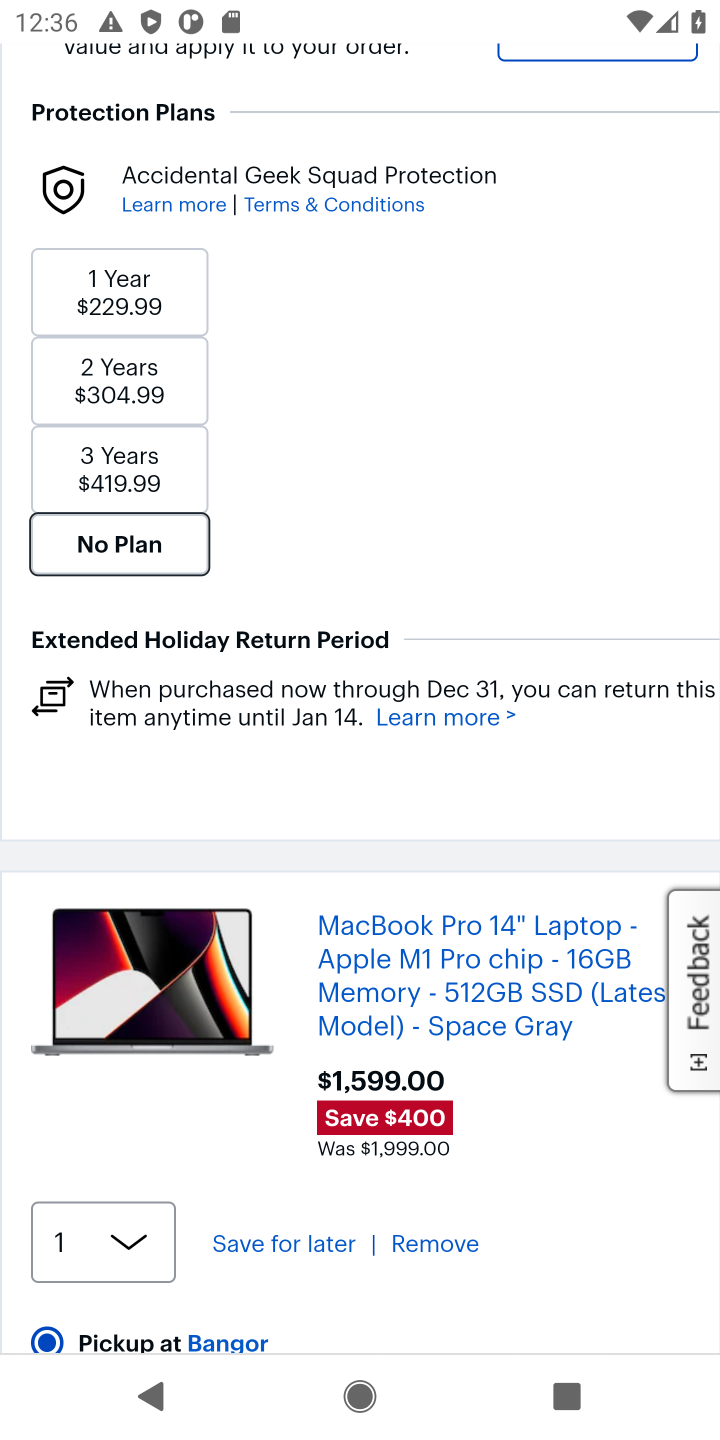
Step 67: click (428, 1243)
Your task to perform on an android device: Add "razer blade" to the cart on bestbuy, then select checkout. Image 68: 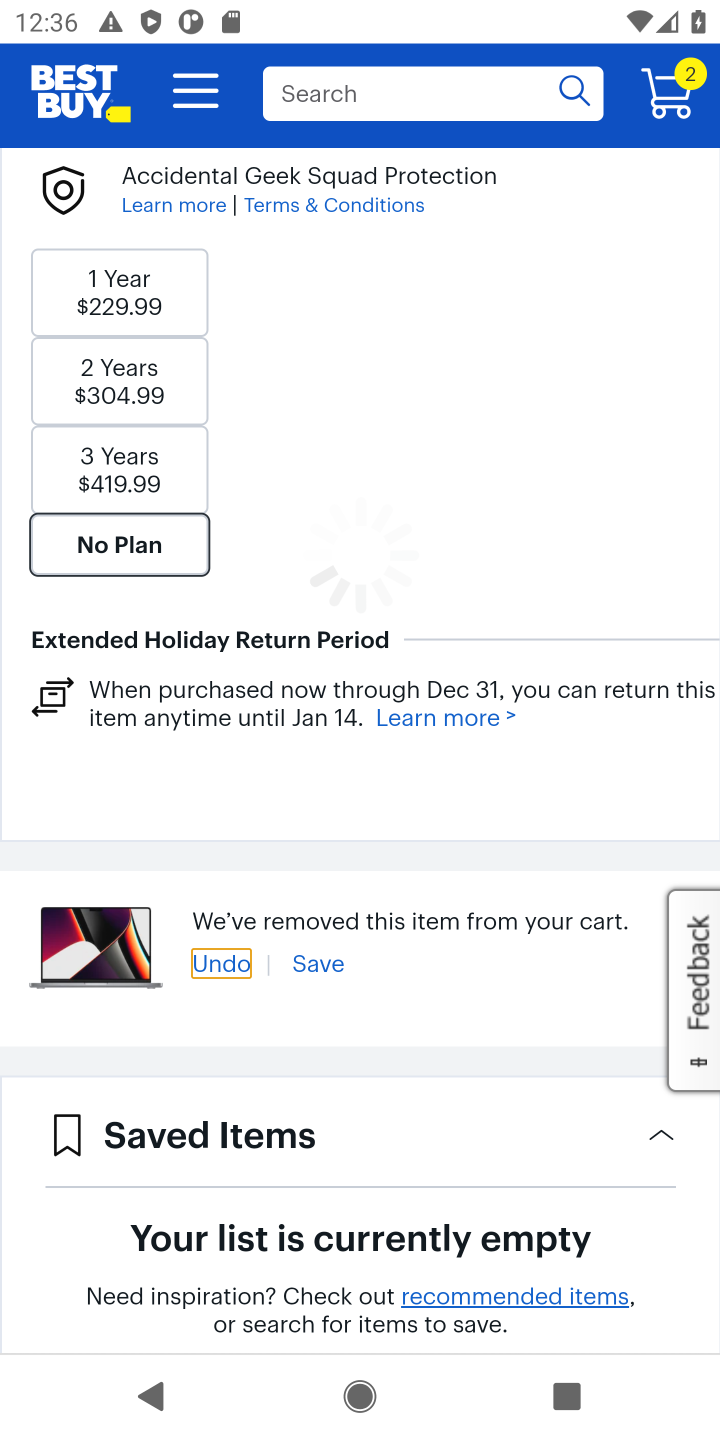
Step 68: drag from (433, 1033) to (378, 1435)
Your task to perform on an android device: Add "razer blade" to the cart on bestbuy, then select checkout. Image 69: 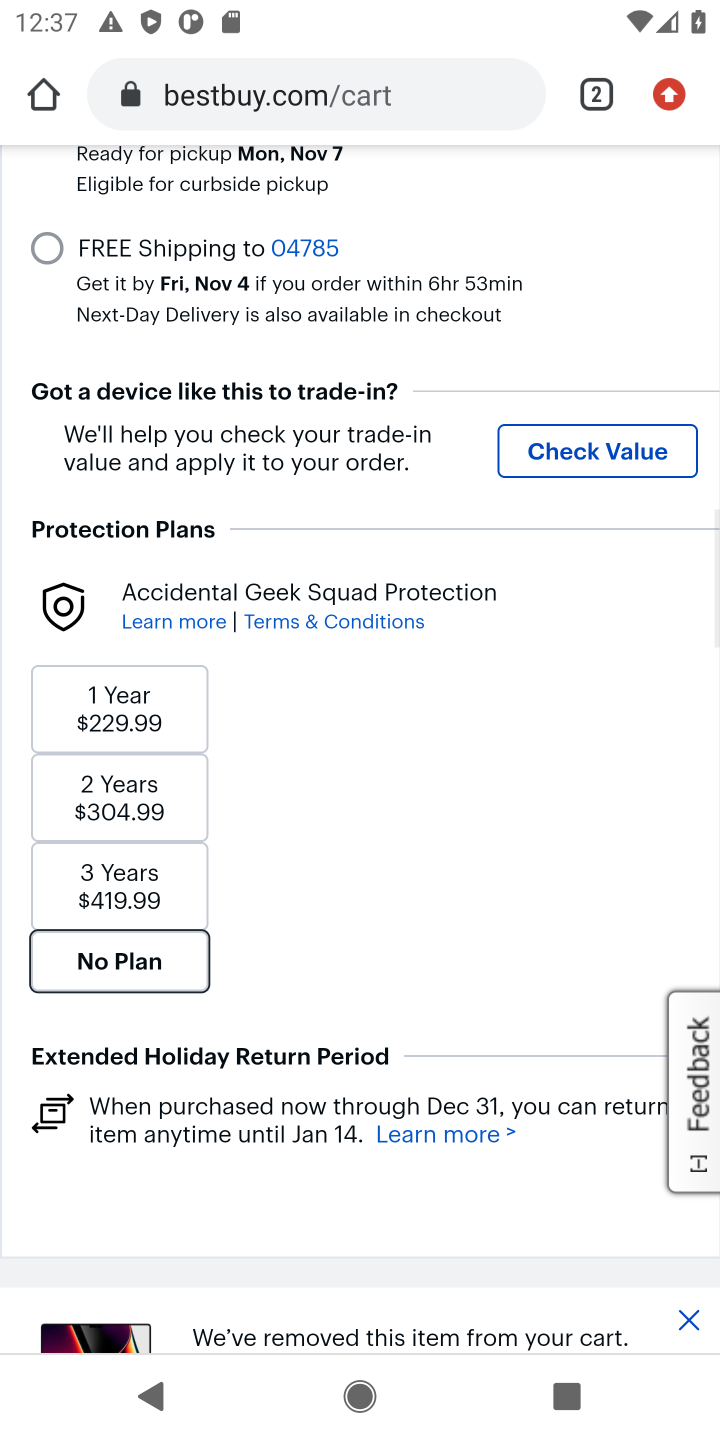
Step 69: drag from (503, 680) to (456, 1392)
Your task to perform on an android device: Add "razer blade" to the cart on bestbuy, then select checkout. Image 70: 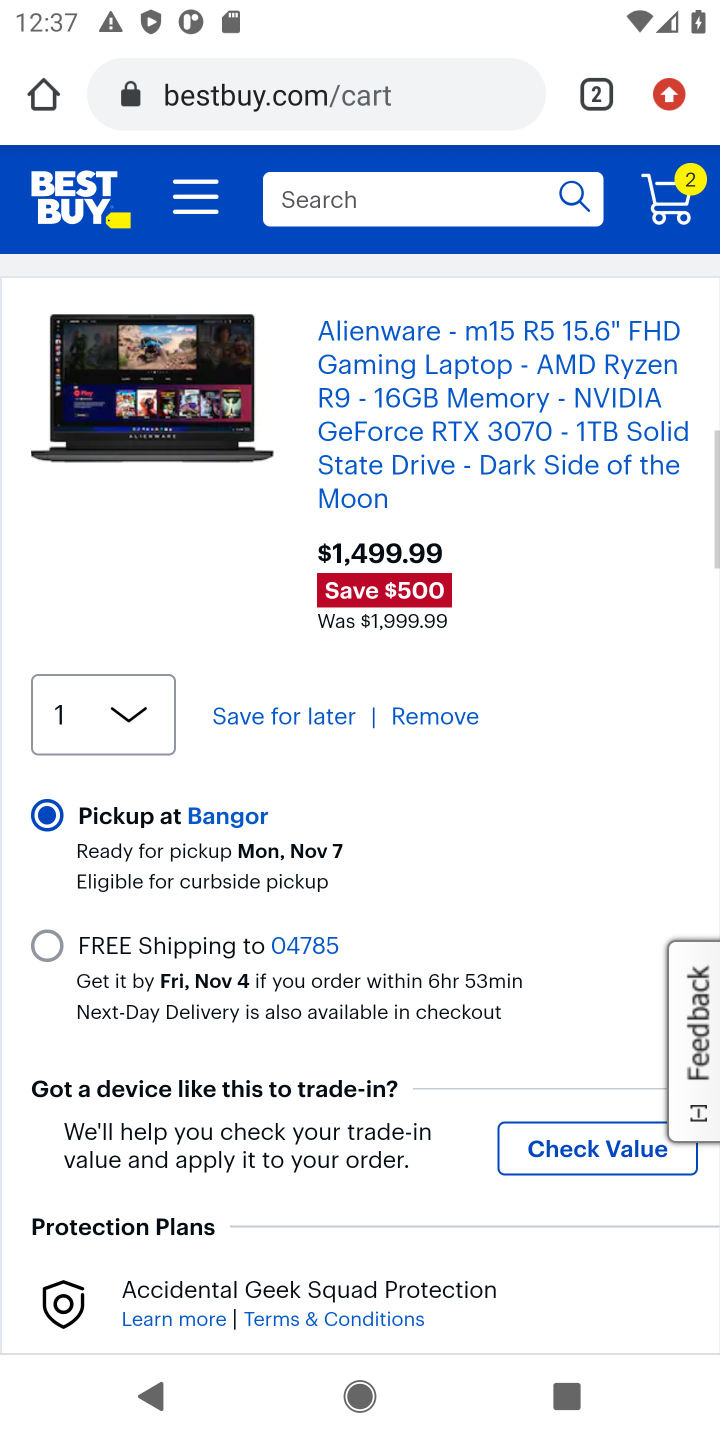
Step 70: drag from (517, 667) to (436, 1260)
Your task to perform on an android device: Add "razer blade" to the cart on bestbuy, then select checkout. Image 71: 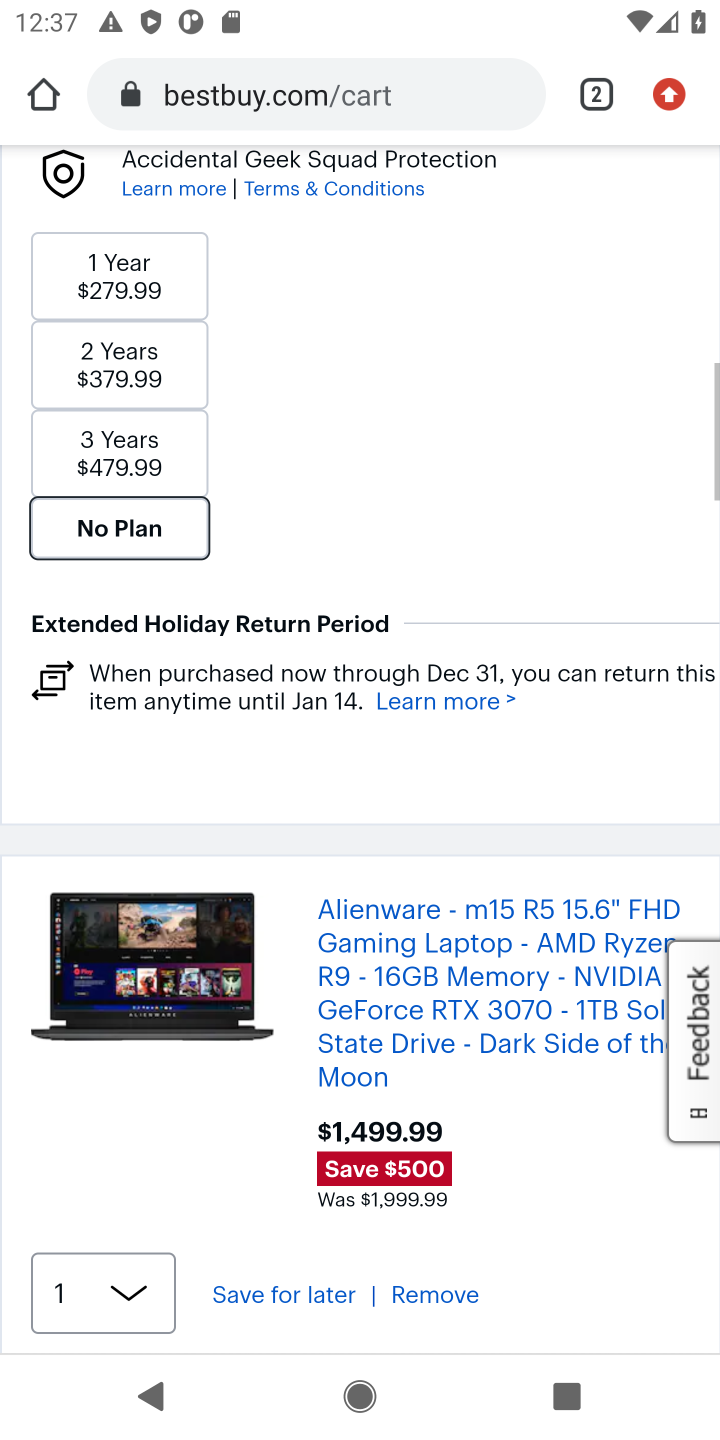
Step 71: drag from (535, 570) to (470, 1127)
Your task to perform on an android device: Add "razer blade" to the cart on bestbuy, then select checkout. Image 72: 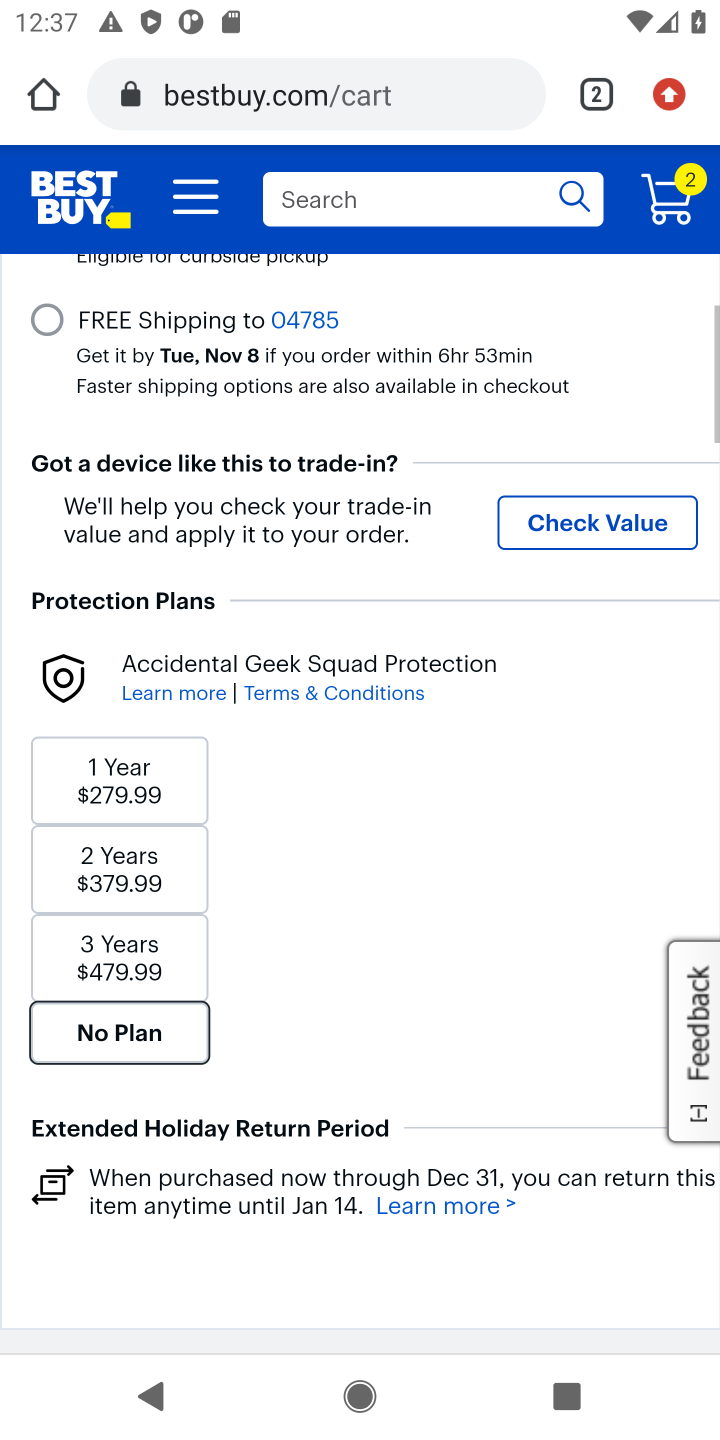
Step 72: drag from (526, 513) to (449, 1030)
Your task to perform on an android device: Add "razer blade" to the cart on bestbuy, then select checkout. Image 73: 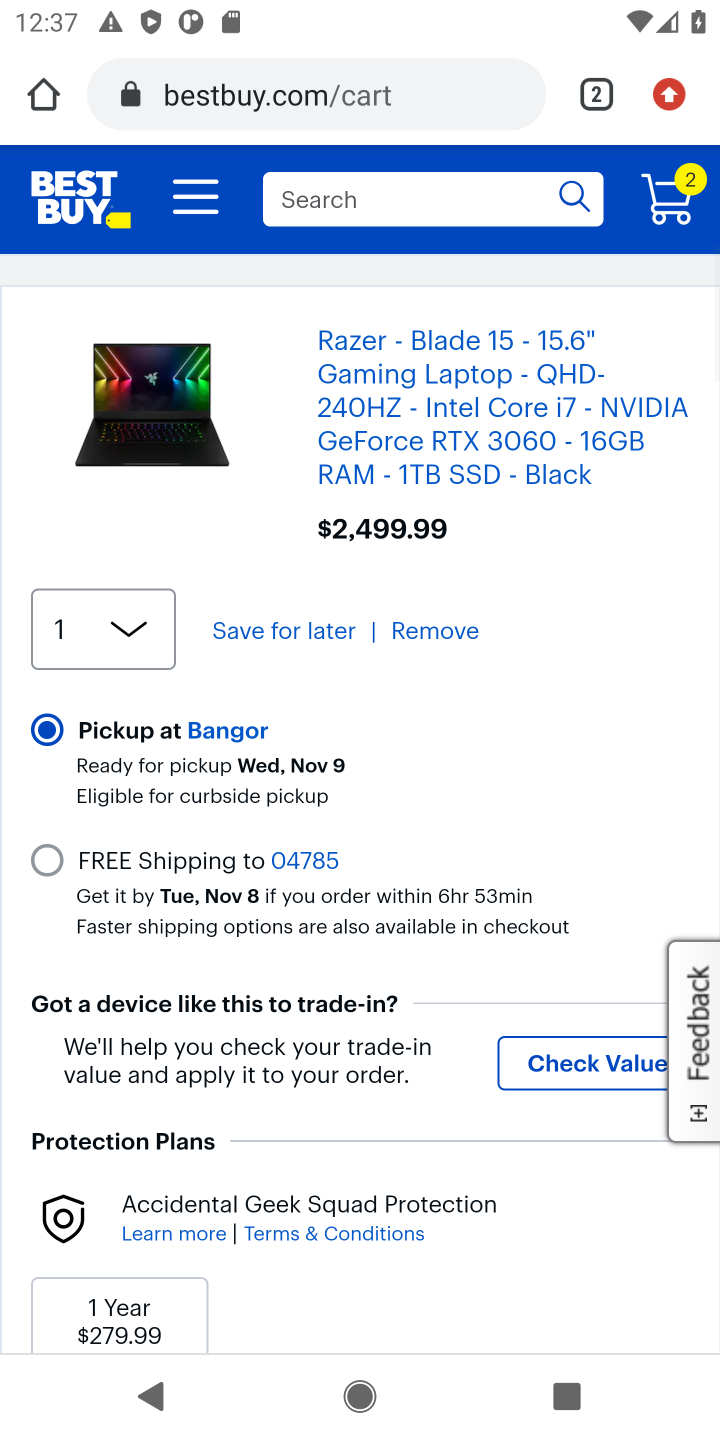
Step 73: drag from (451, 553) to (417, 1177)
Your task to perform on an android device: Add "razer blade" to the cart on bestbuy, then select checkout. Image 74: 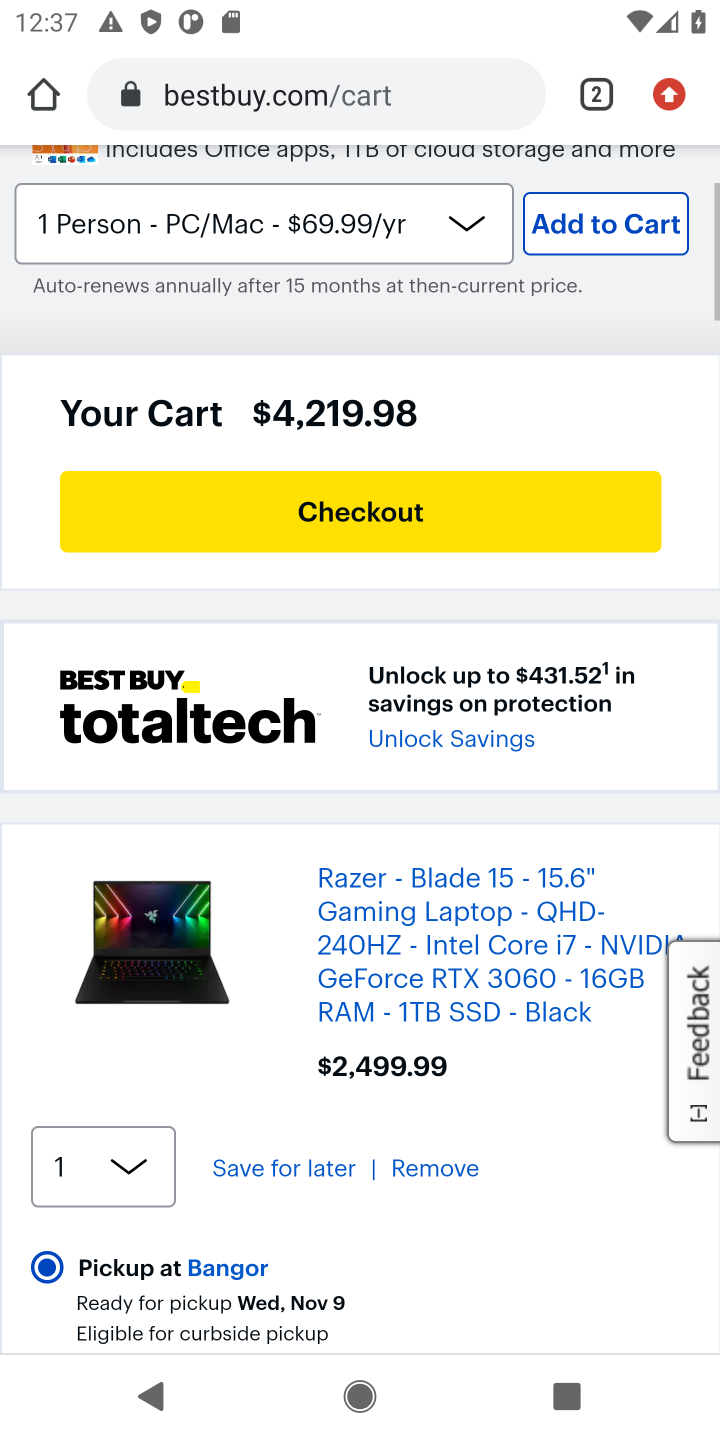
Step 74: click (427, 441)
Your task to perform on an android device: Add "razer blade" to the cart on bestbuy, then select checkout. Image 75: 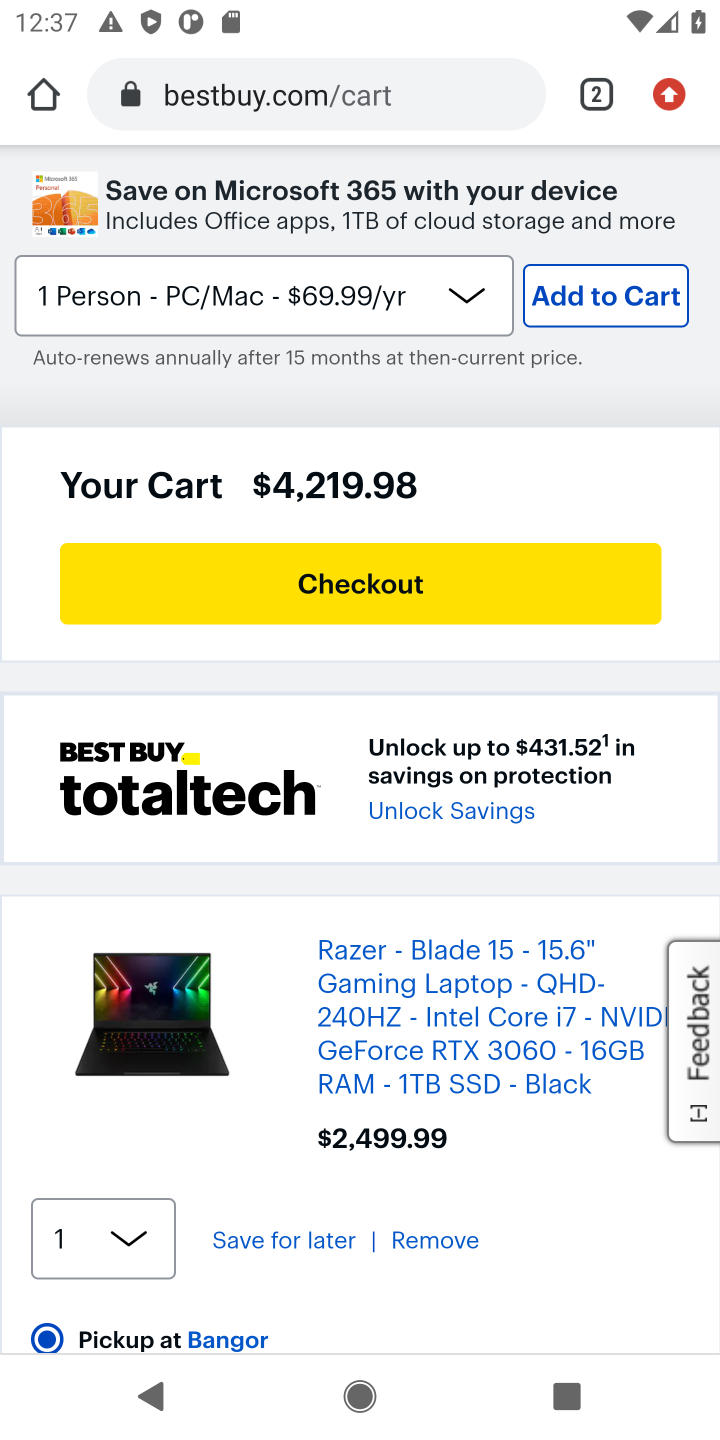
Step 75: click (408, 508)
Your task to perform on an android device: Add "razer blade" to the cart on bestbuy, then select checkout. Image 76: 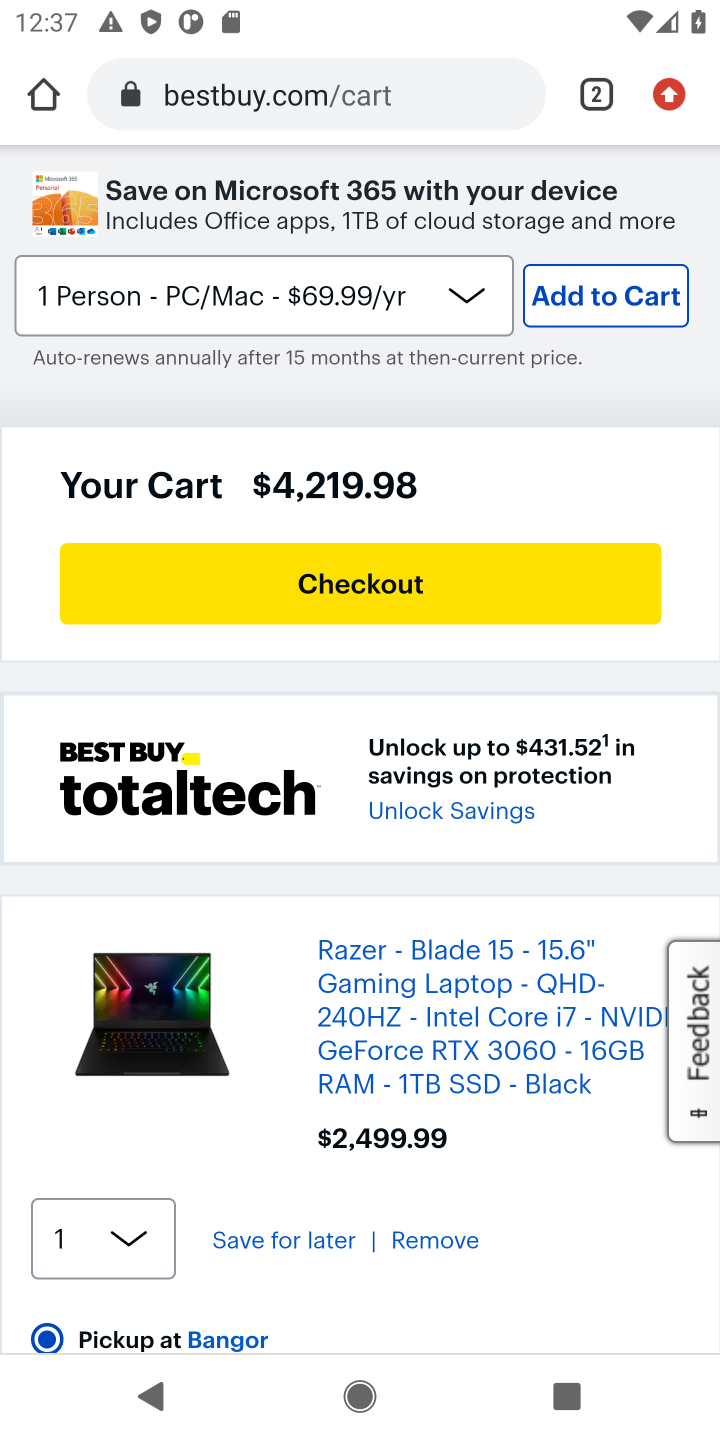
Step 76: click (408, 565)
Your task to perform on an android device: Add "razer blade" to the cart on bestbuy, then select checkout. Image 77: 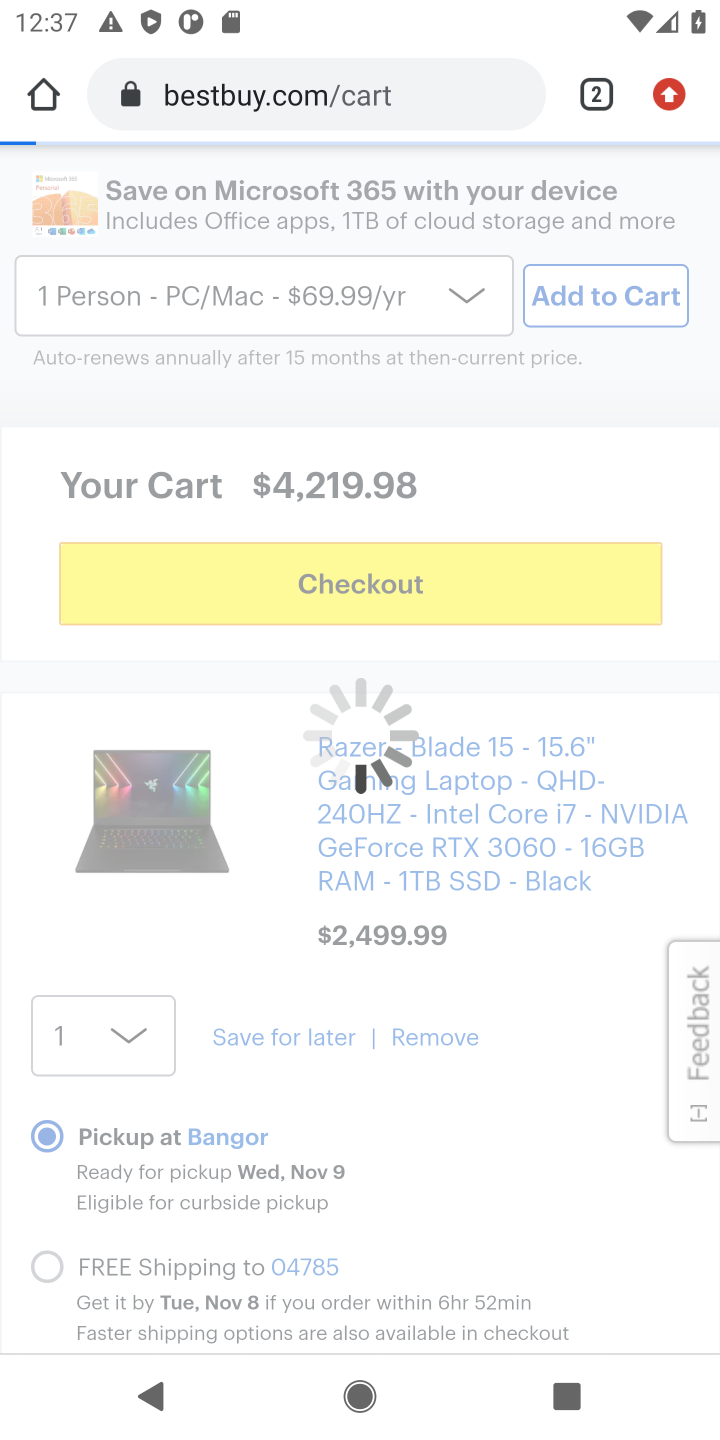
Step 77: task complete